Your task to perform on an android device: What's the news in theFalkland Islands? Image 0: 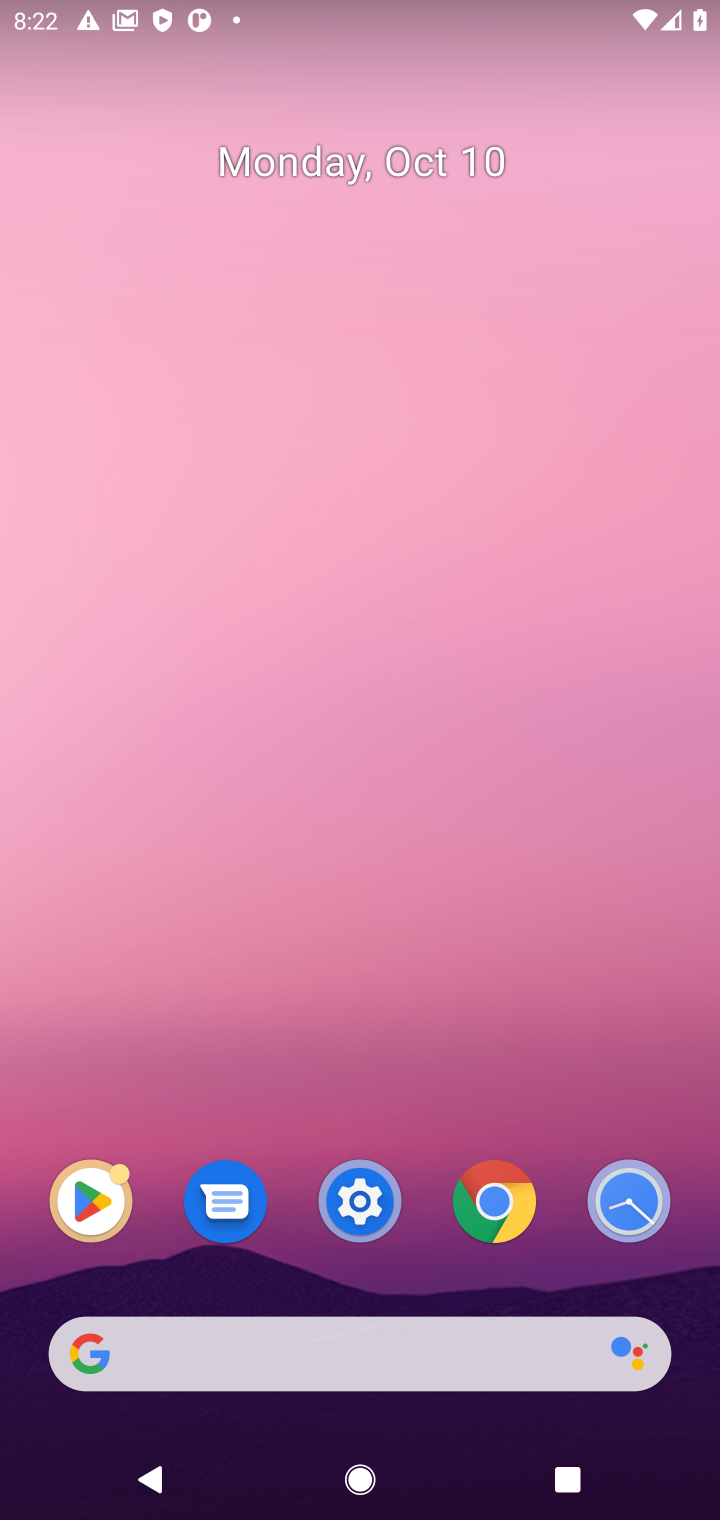
Step 0: click (474, 1193)
Your task to perform on an android device: What's the news in theFalkland Islands? Image 1: 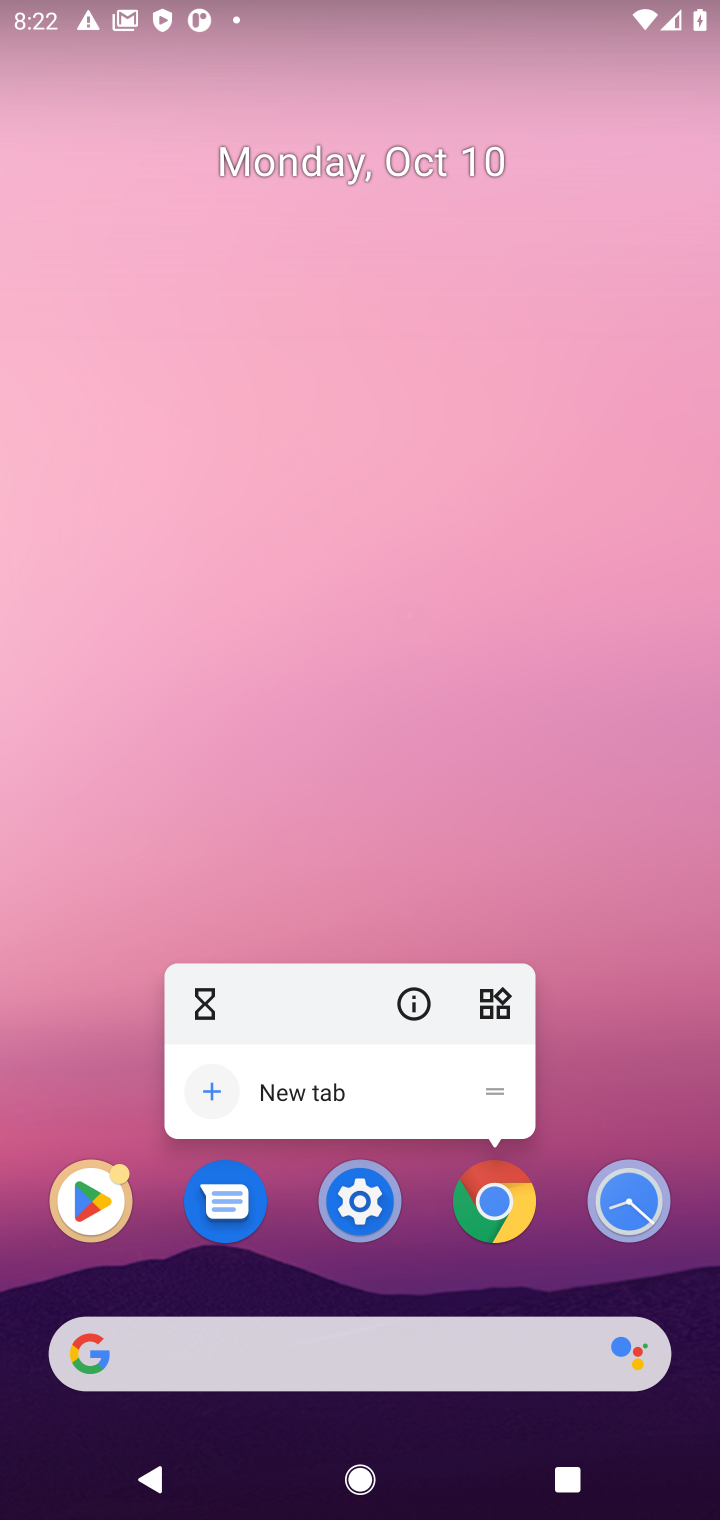
Step 1: click (490, 1201)
Your task to perform on an android device: What's the news in theFalkland Islands? Image 2: 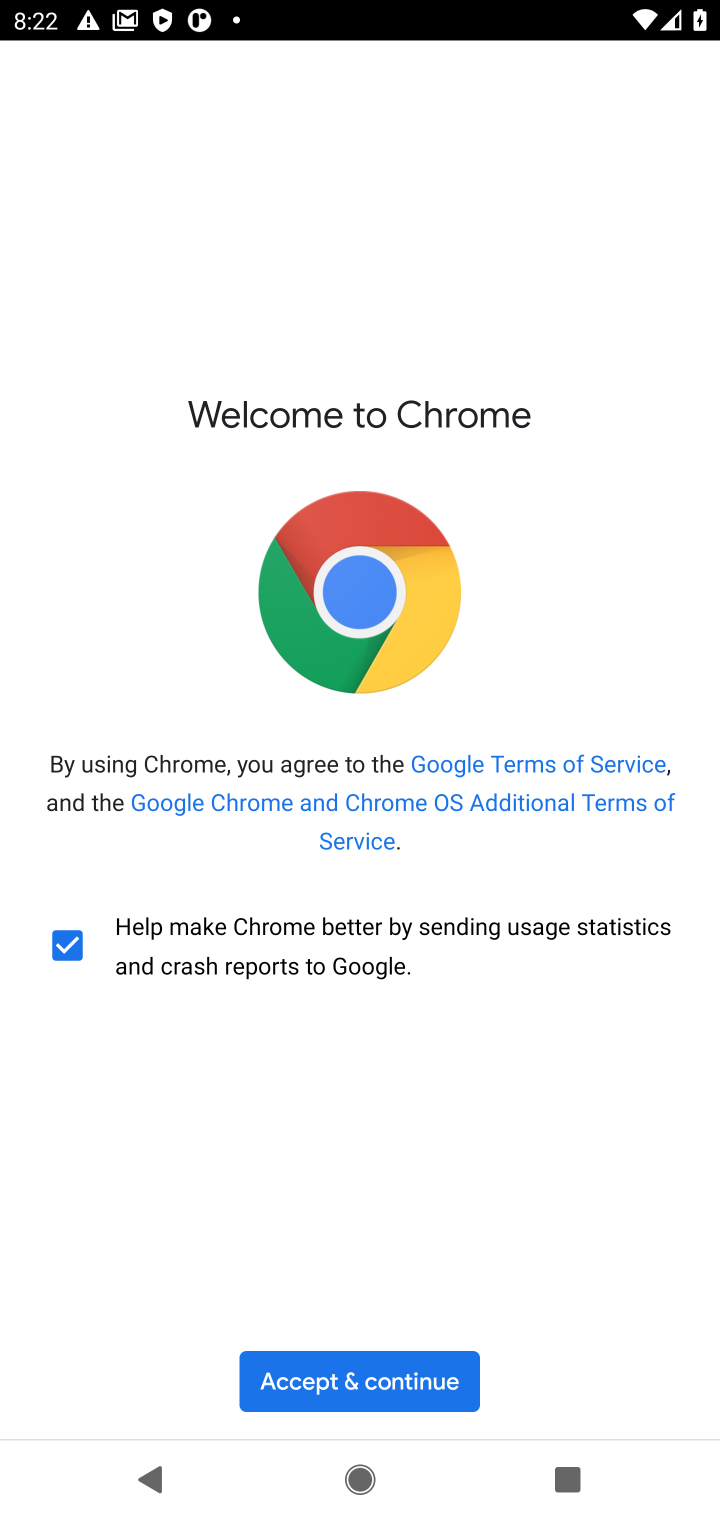
Step 2: click (368, 1375)
Your task to perform on an android device: What's the news in theFalkland Islands? Image 3: 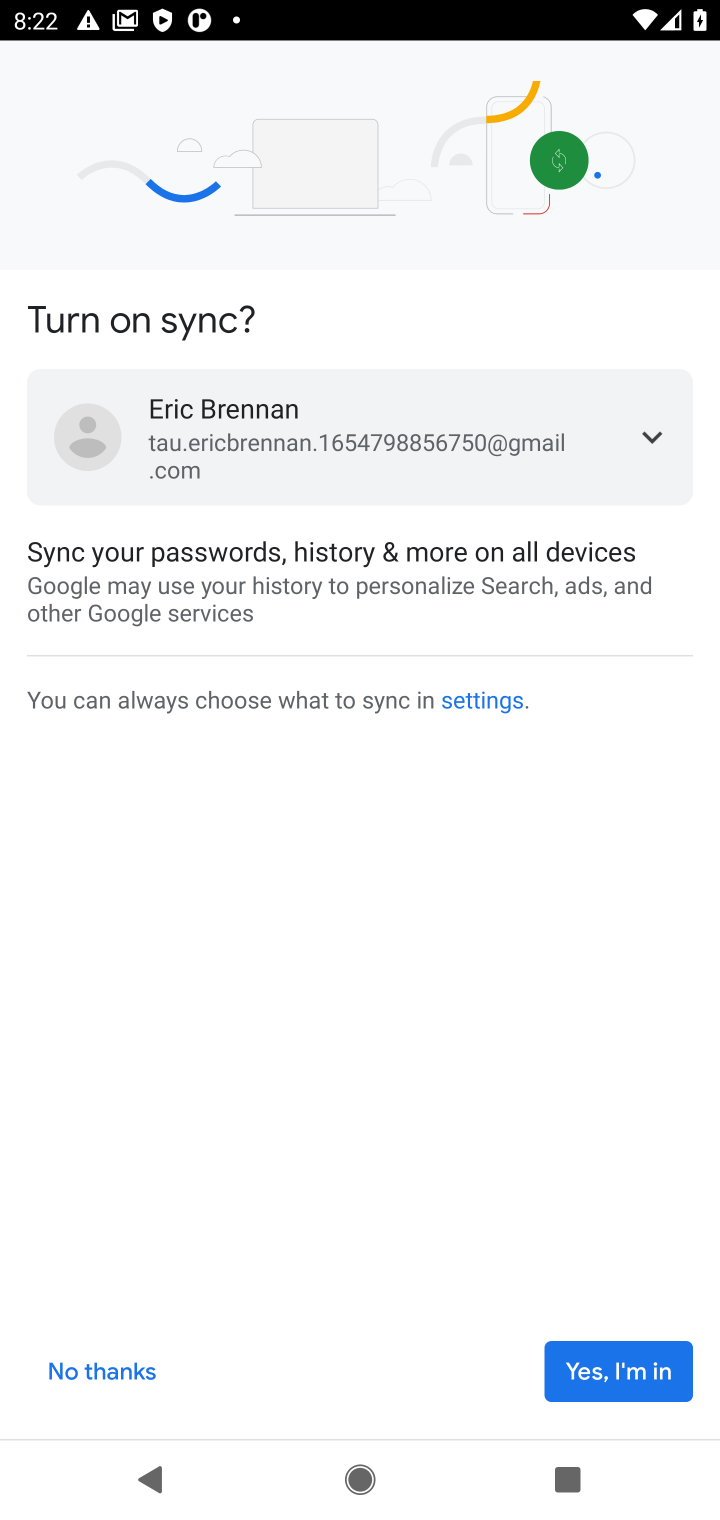
Step 3: click (550, 1349)
Your task to perform on an android device: What's the news in theFalkland Islands? Image 4: 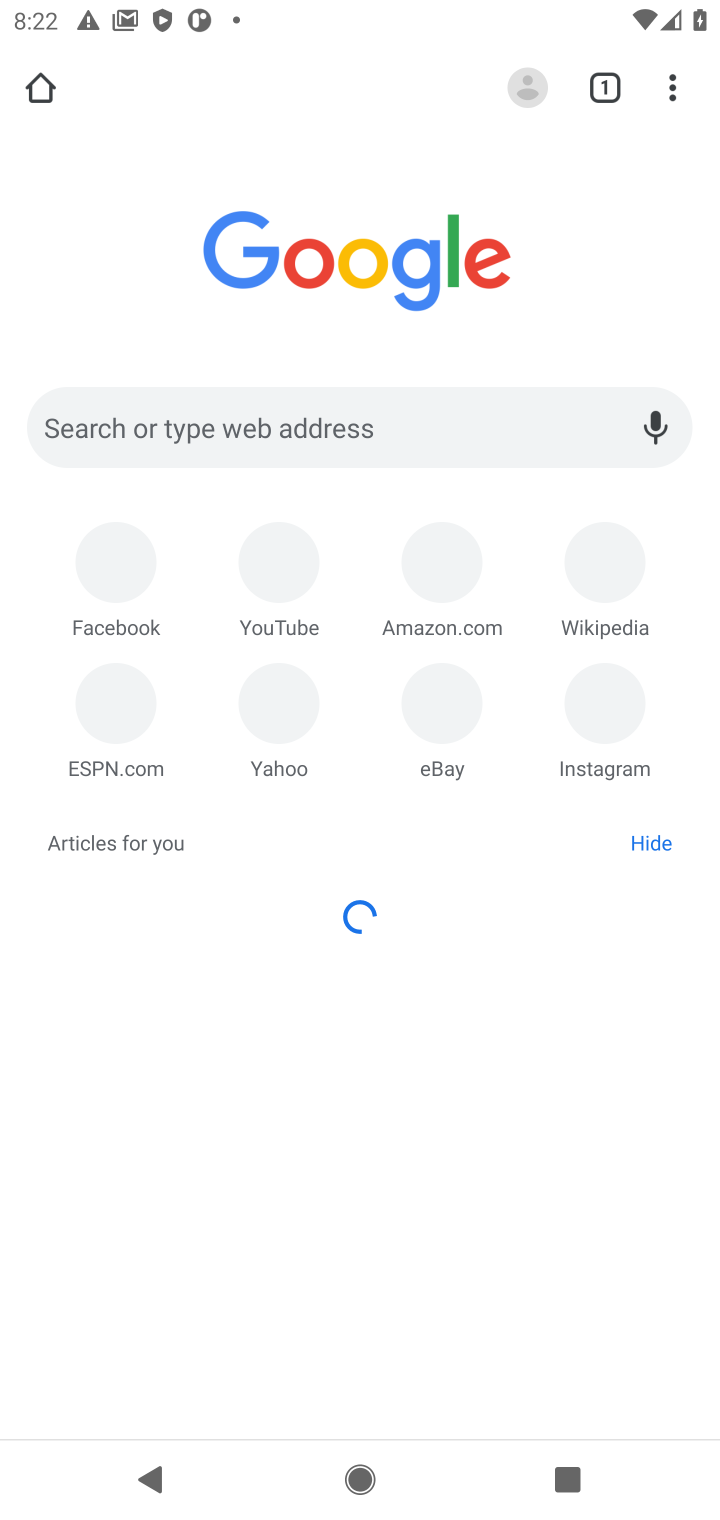
Step 4: click (197, 433)
Your task to perform on an android device: What's the news in theFalkland Islands? Image 5: 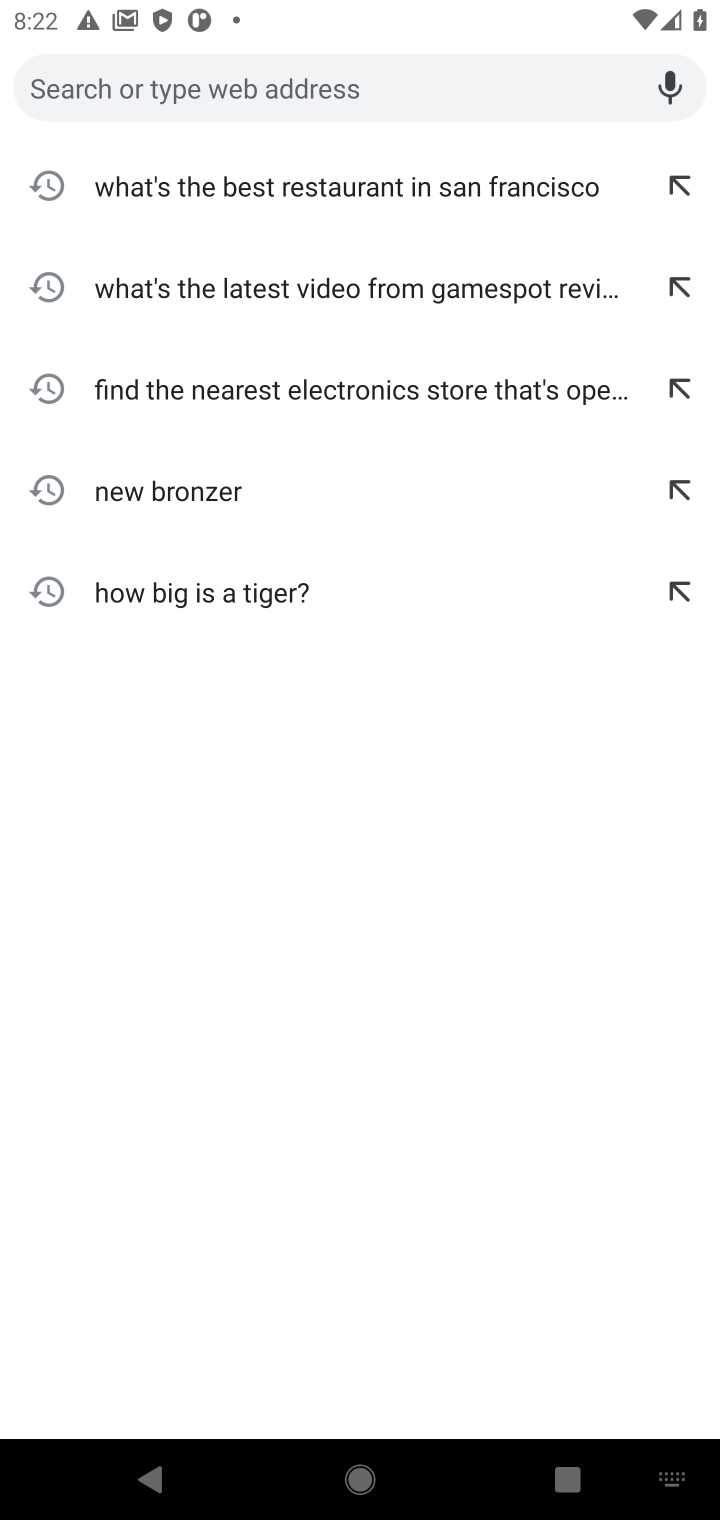
Step 5: type "What's the news in theFalkland Islands?"
Your task to perform on an android device: What's the news in theFalkland Islands? Image 6: 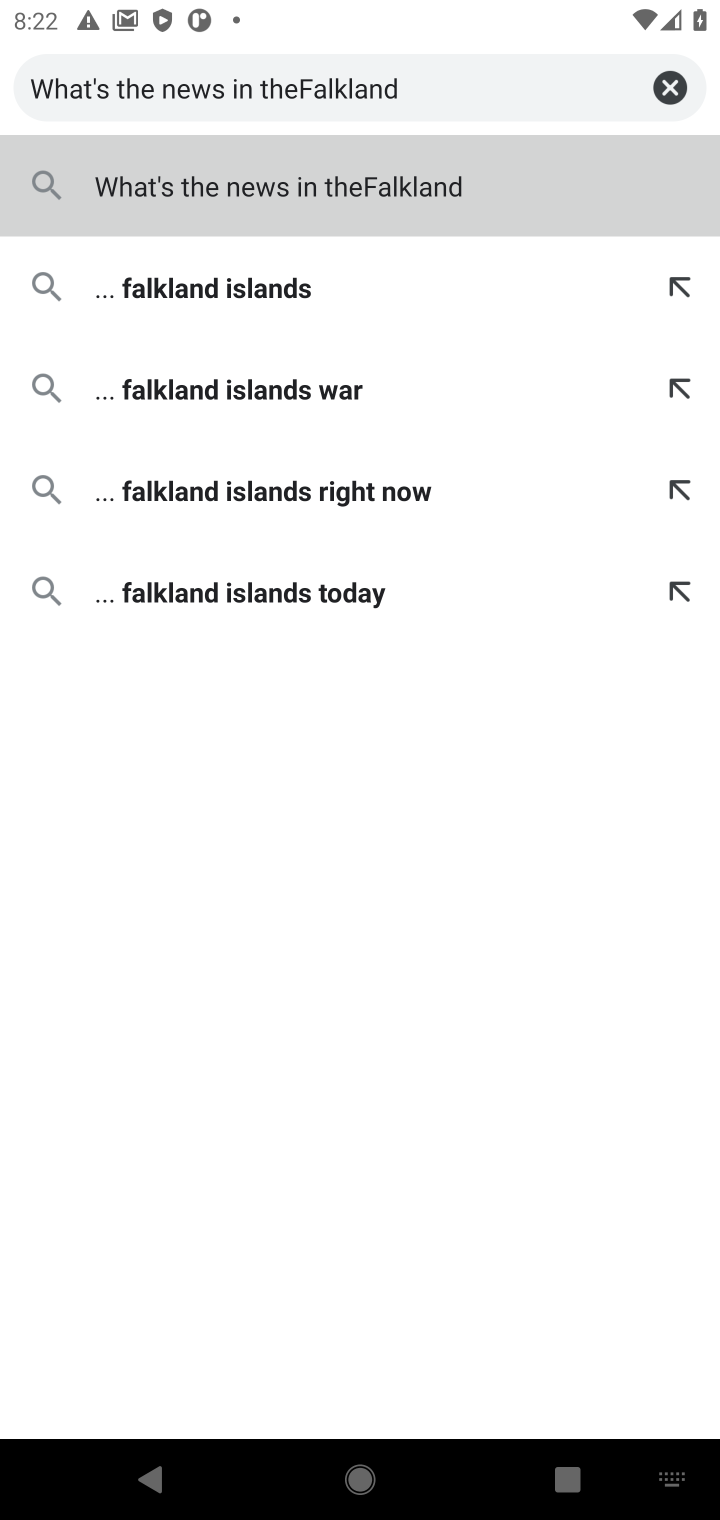
Step 6: type ""
Your task to perform on an android device: What's the news in theFalkland Islands? Image 7: 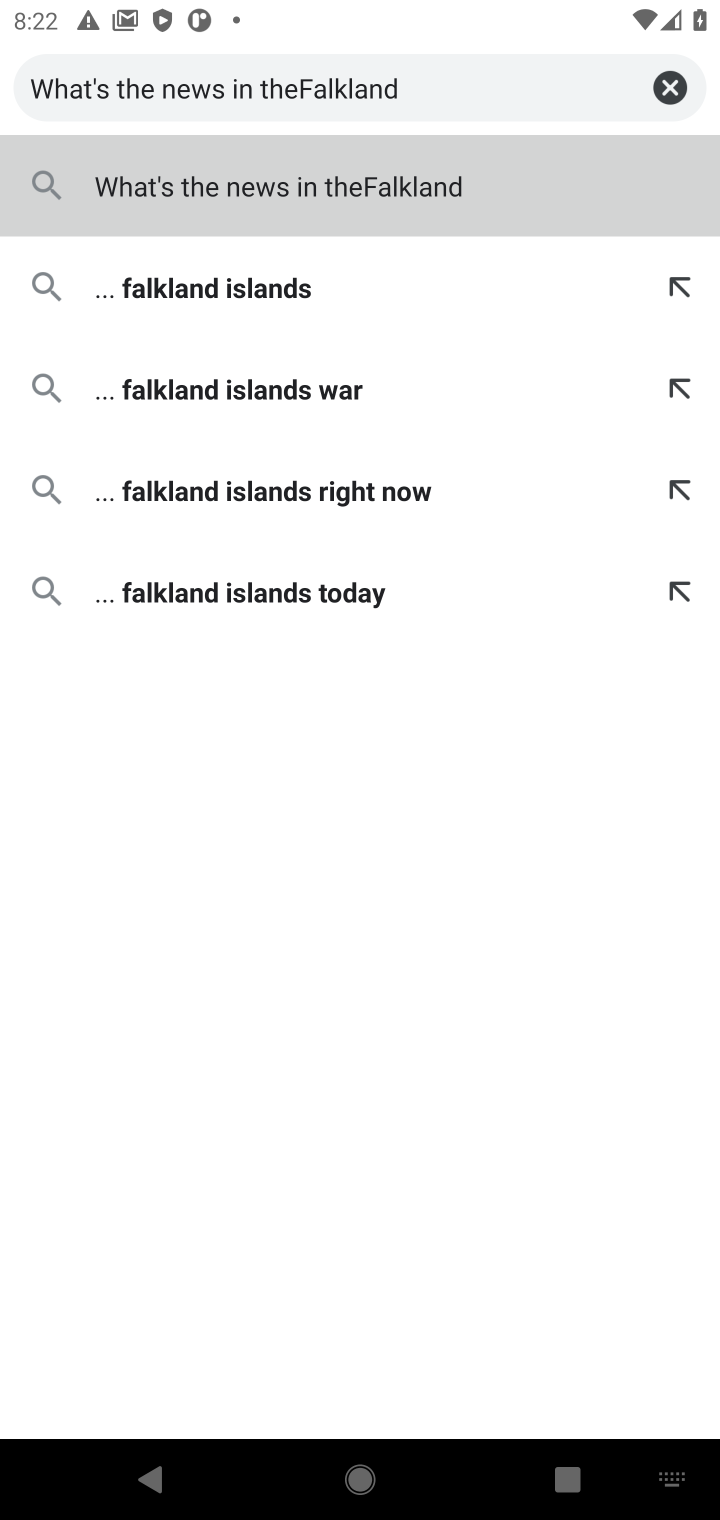
Step 7: click (369, 185)
Your task to perform on an android device: What's the news in theFalkland Islands? Image 8: 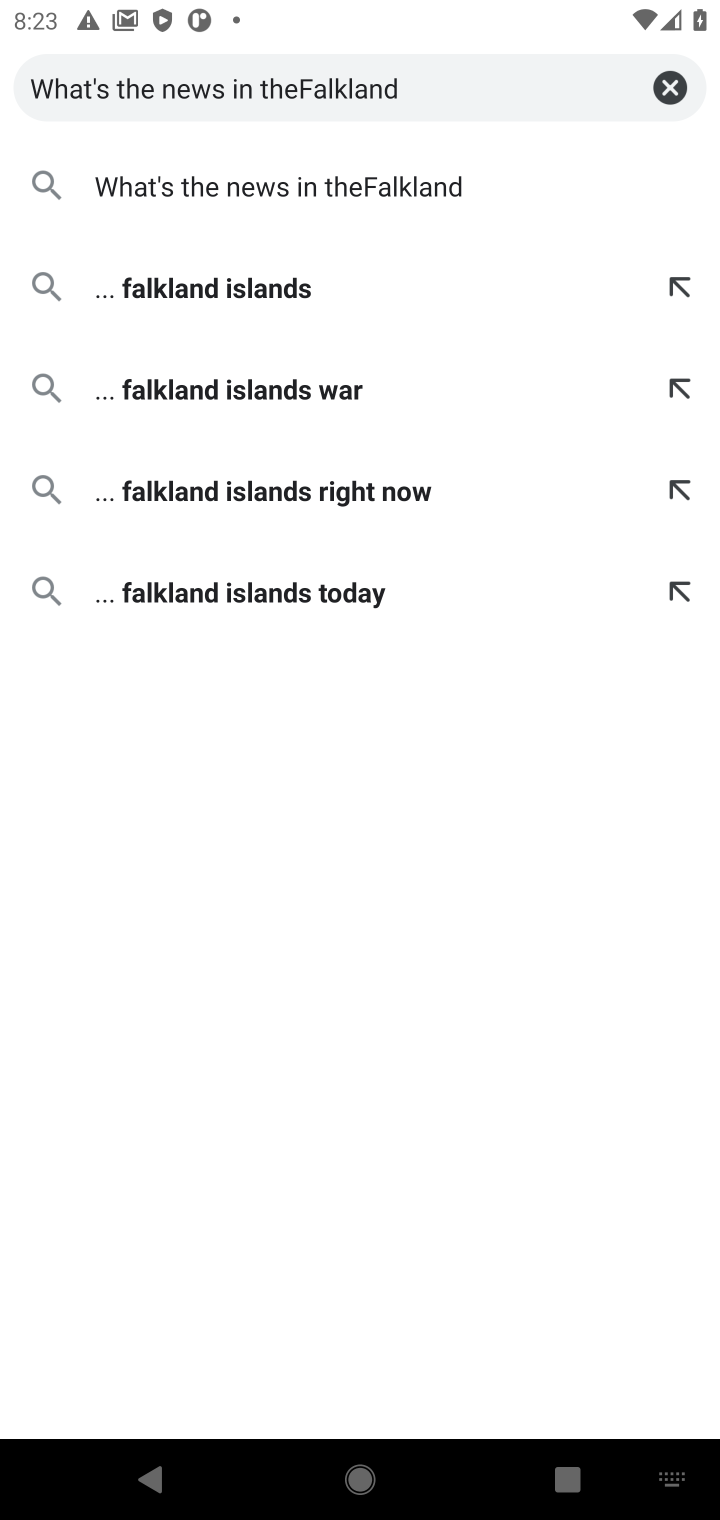
Step 8: click (369, 185)
Your task to perform on an android device: What's the news in theFalkland Islands? Image 9: 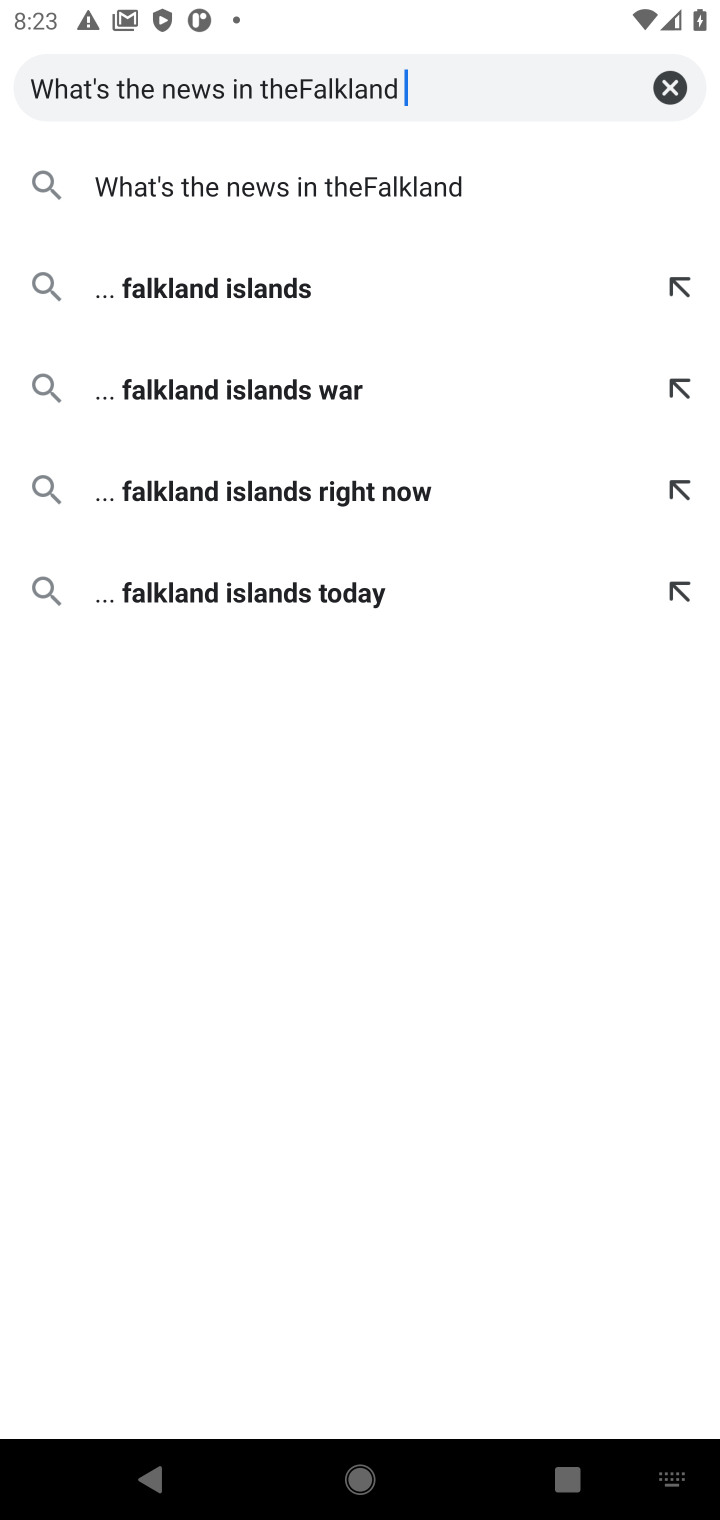
Step 9: press enter
Your task to perform on an android device: What's the news in theFalkland Islands? Image 10: 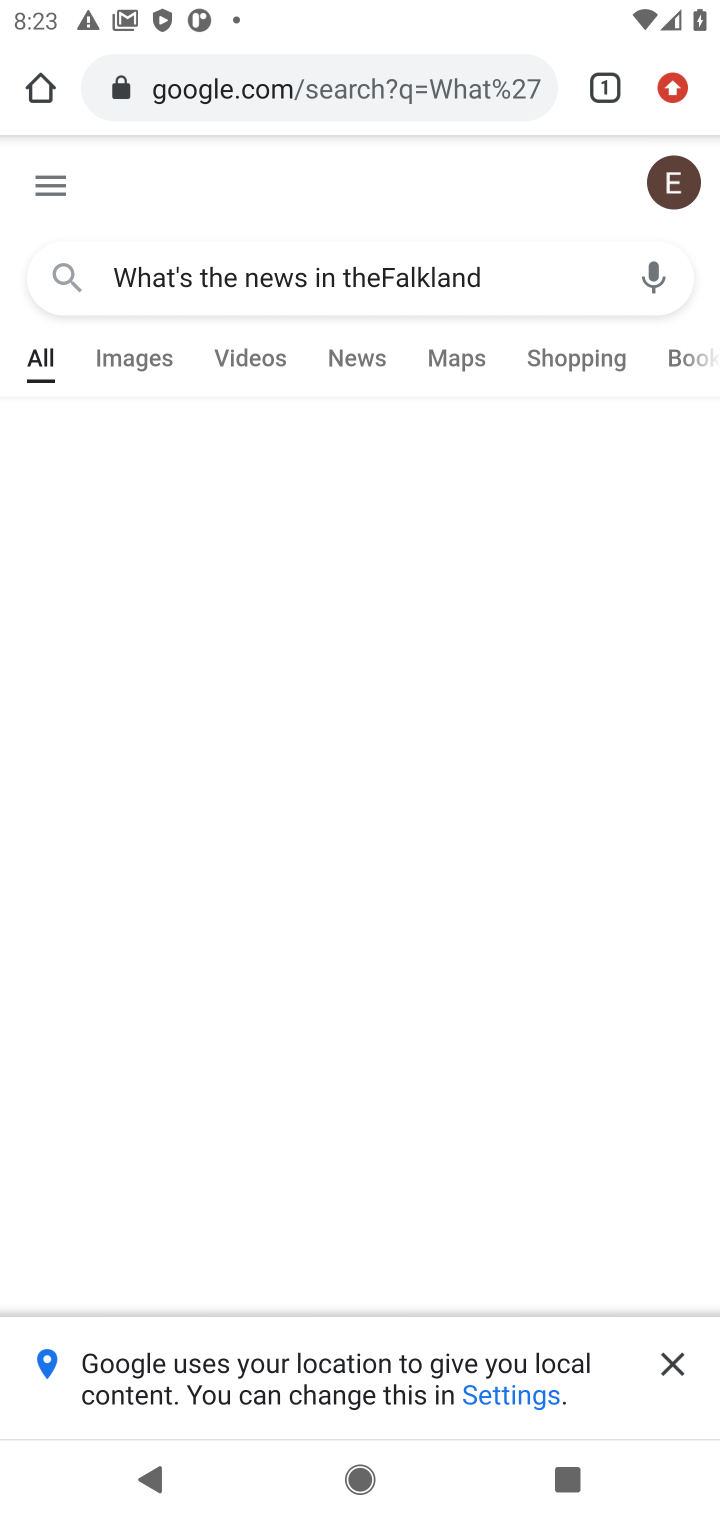
Step 10: click (669, 1370)
Your task to perform on an android device: What's the news in theFalkland Islands? Image 11: 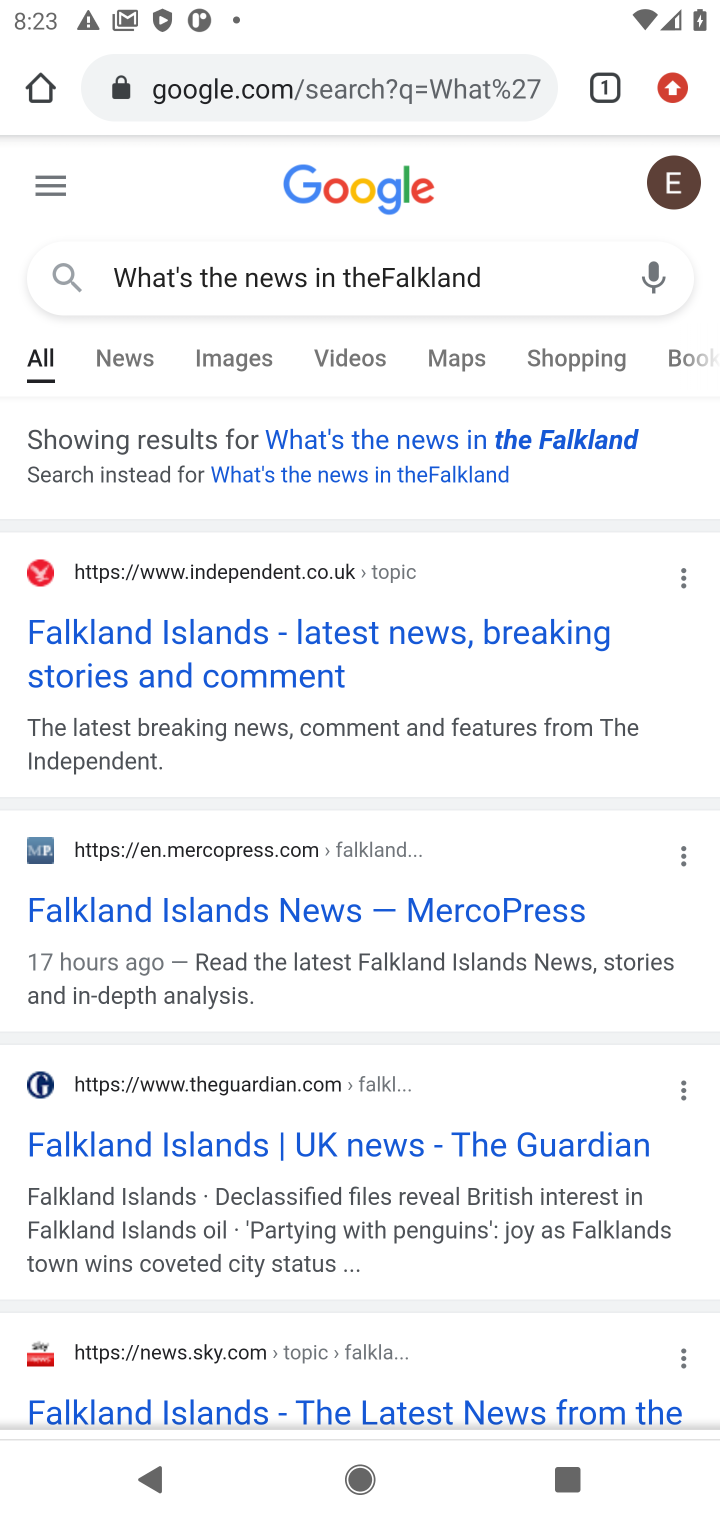
Step 11: drag from (336, 1180) to (460, 289)
Your task to perform on an android device: What's the news in theFalkland Islands? Image 12: 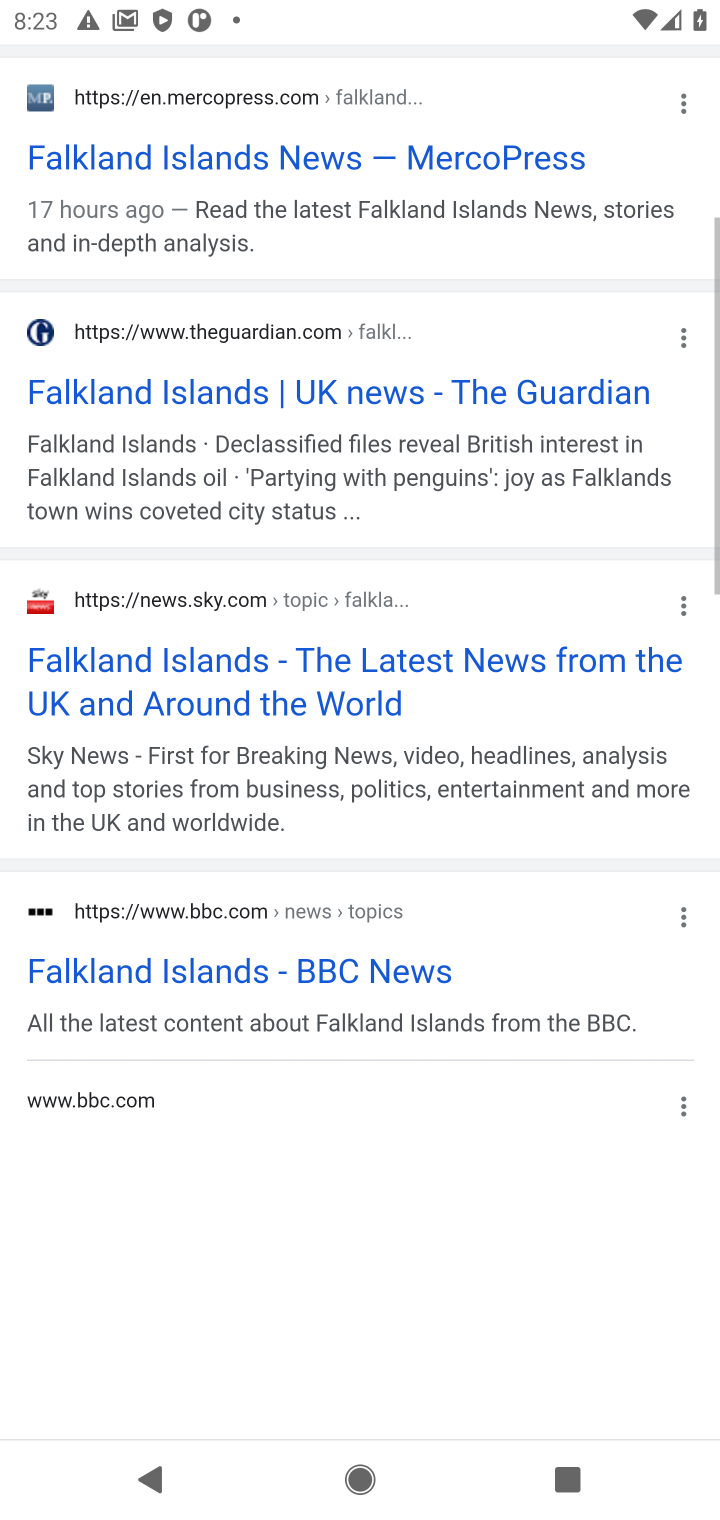
Step 12: drag from (228, 831) to (306, 476)
Your task to perform on an android device: What's the news in theFalkland Islands? Image 13: 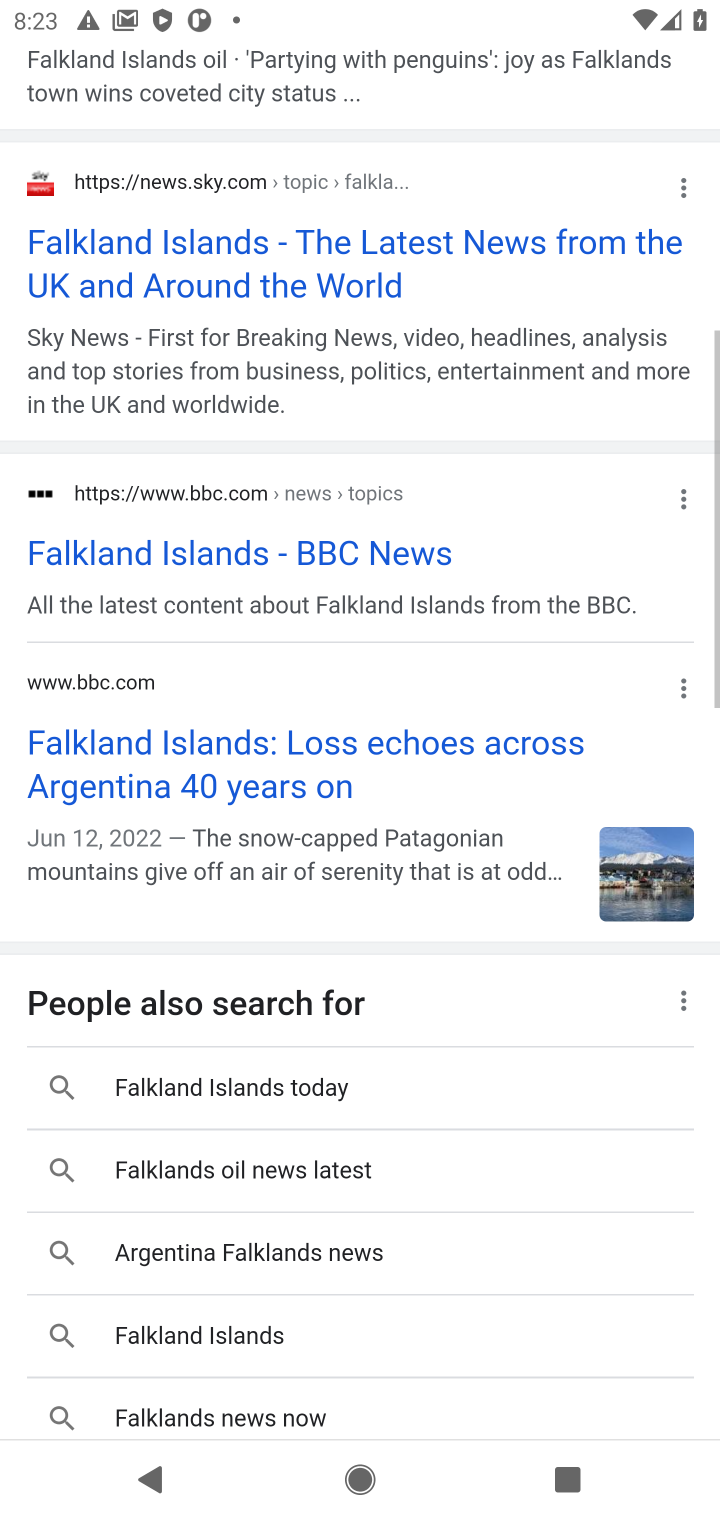
Step 13: drag from (358, 744) to (334, 1272)
Your task to perform on an android device: What's the news in theFalkland Islands? Image 14: 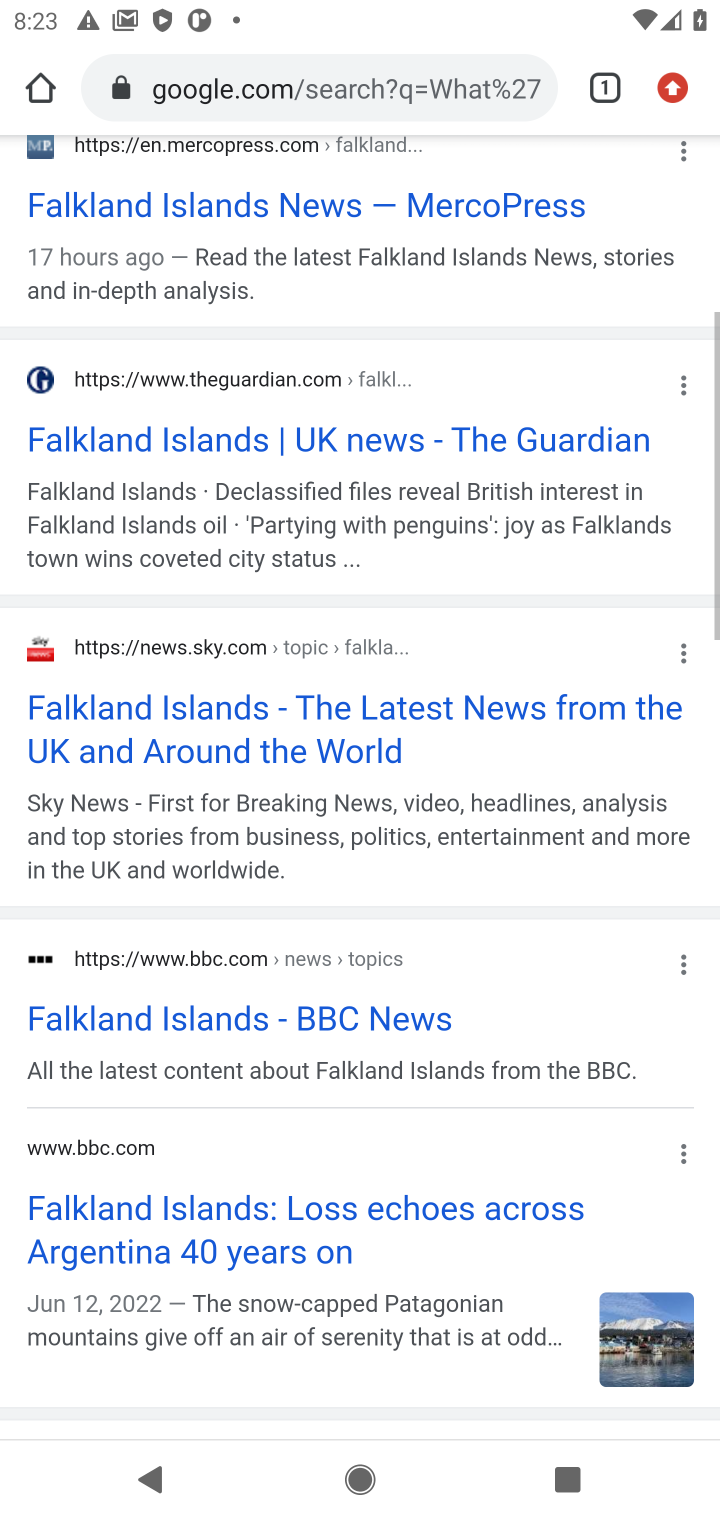
Step 14: drag from (373, 1301) to (373, 1373)
Your task to perform on an android device: What's the news in theFalkland Islands? Image 15: 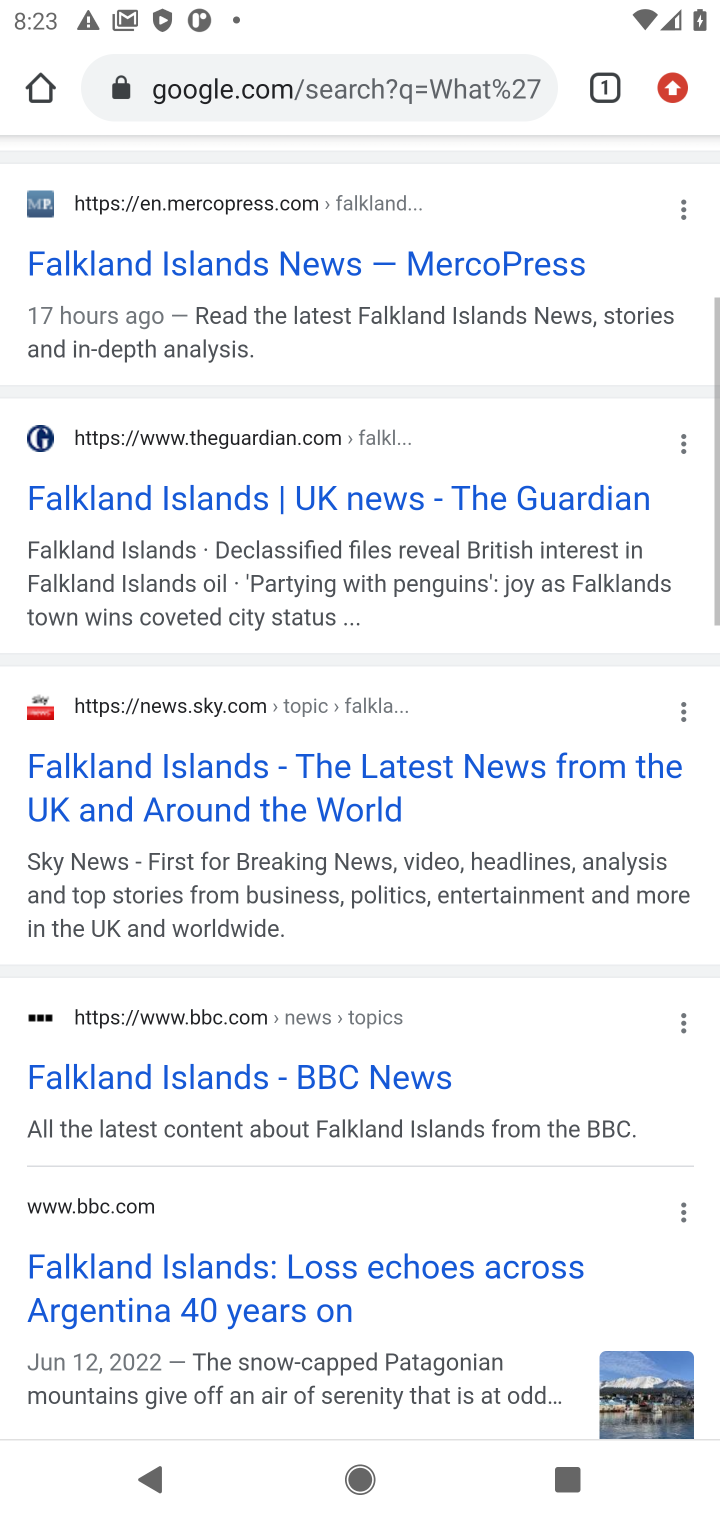
Step 15: click (401, 1296)
Your task to perform on an android device: What's the news in theFalkland Islands? Image 16: 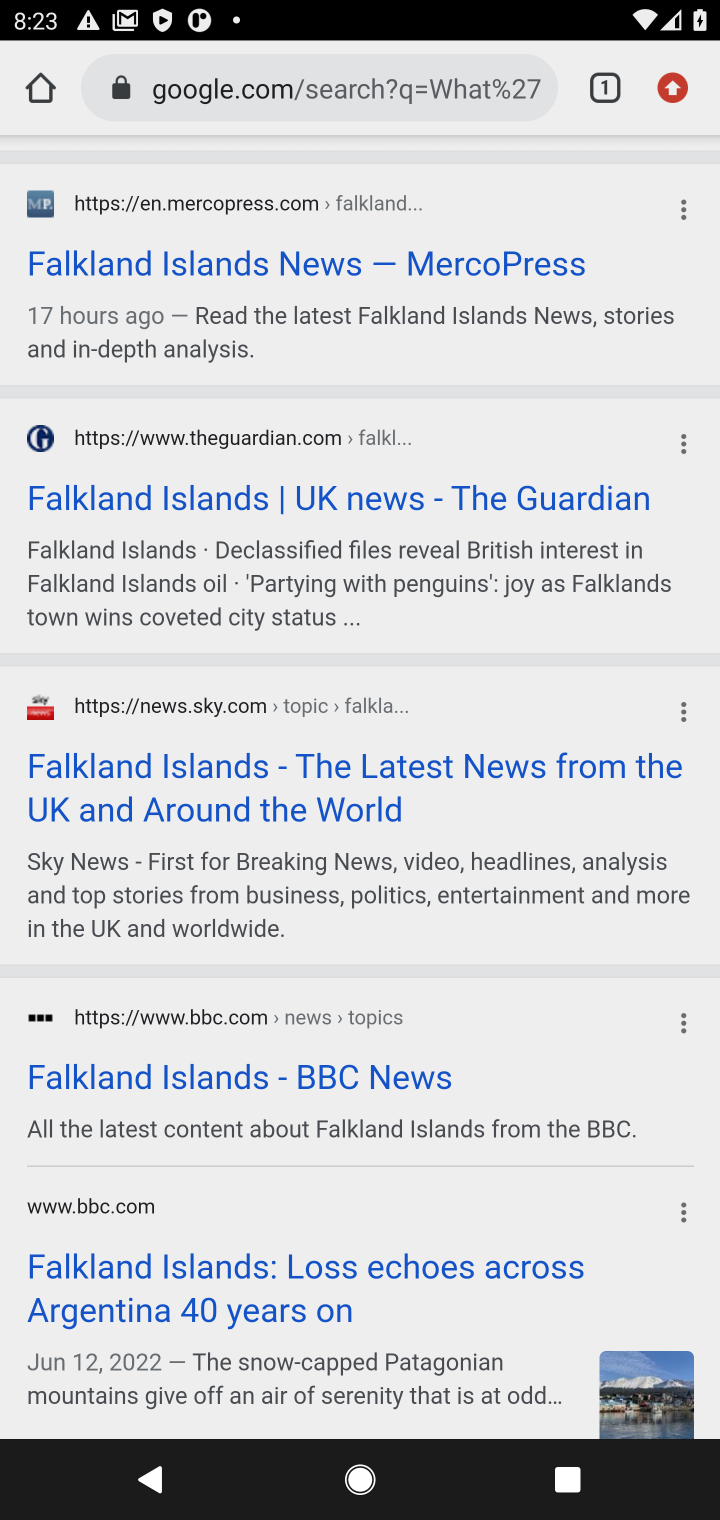
Step 16: click (204, 488)
Your task to perform on an android device: What's the news in theFalkland Islands? Image 17: 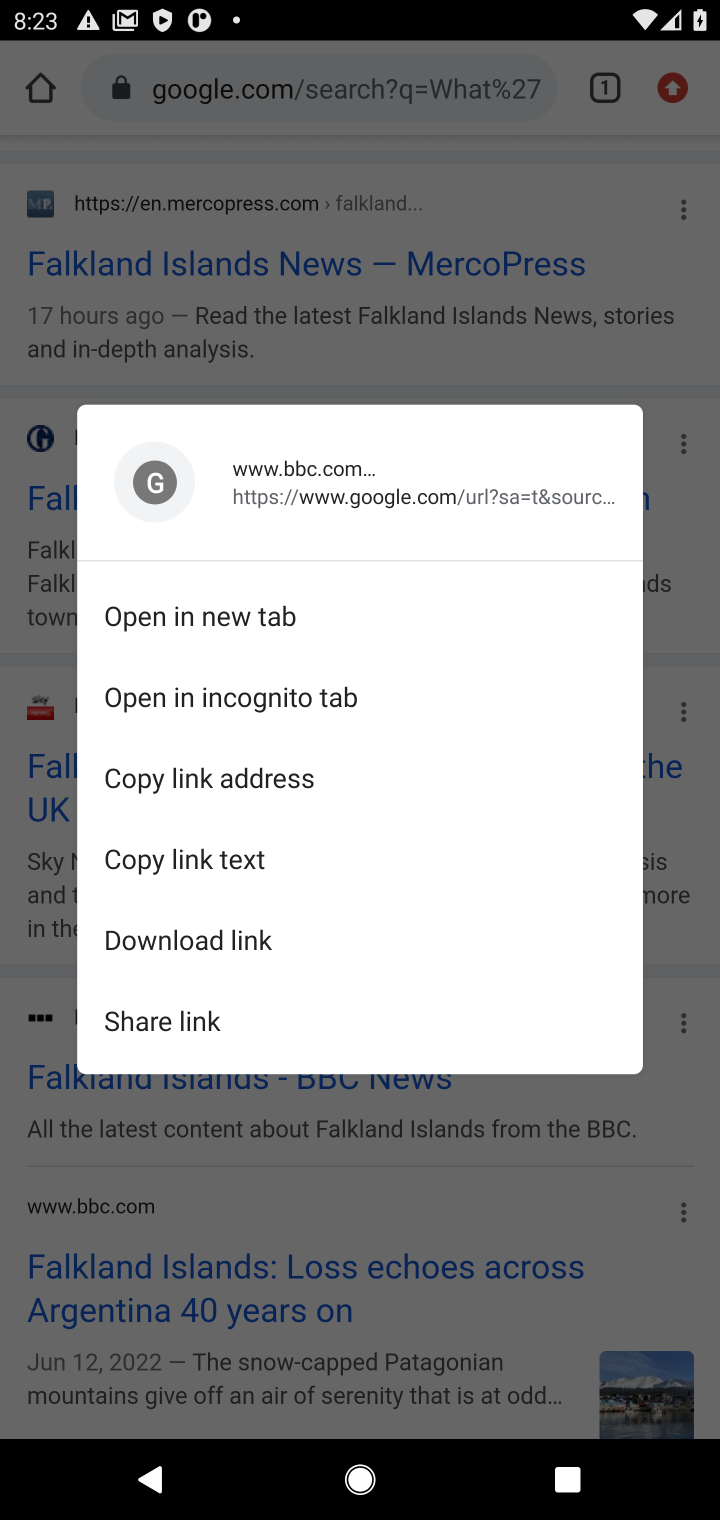
Step 17: click (272, 339)
Your task to perform on an android device: What's the news in theFalkland Islands? Image 18: 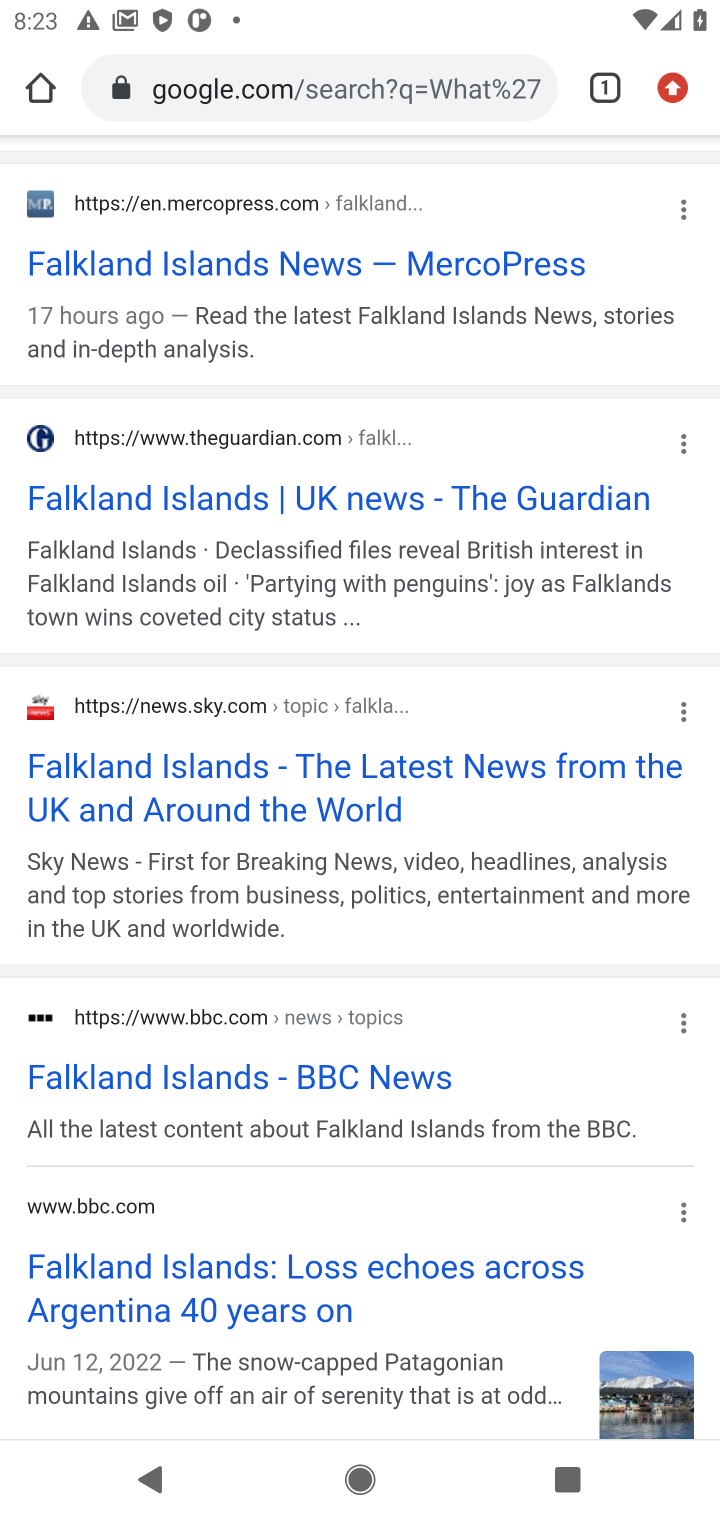
Step 18: click (214, 504)
Your task to perform on an android device: What's the news in theFalkland Islands? Image 19: 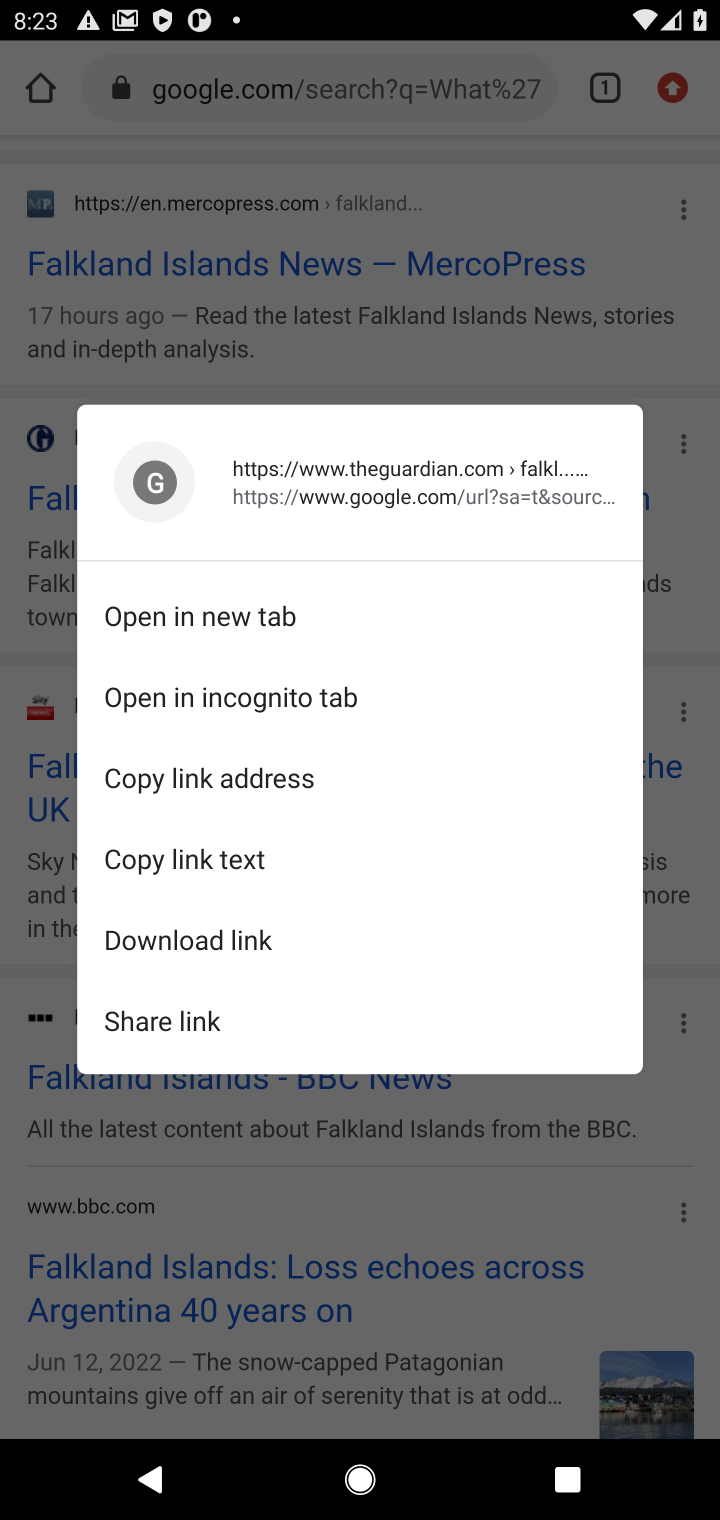
Step 19: click (339, 279)
Your task to perform on an android device: What's the news in theFalkland Islands? Image 20: 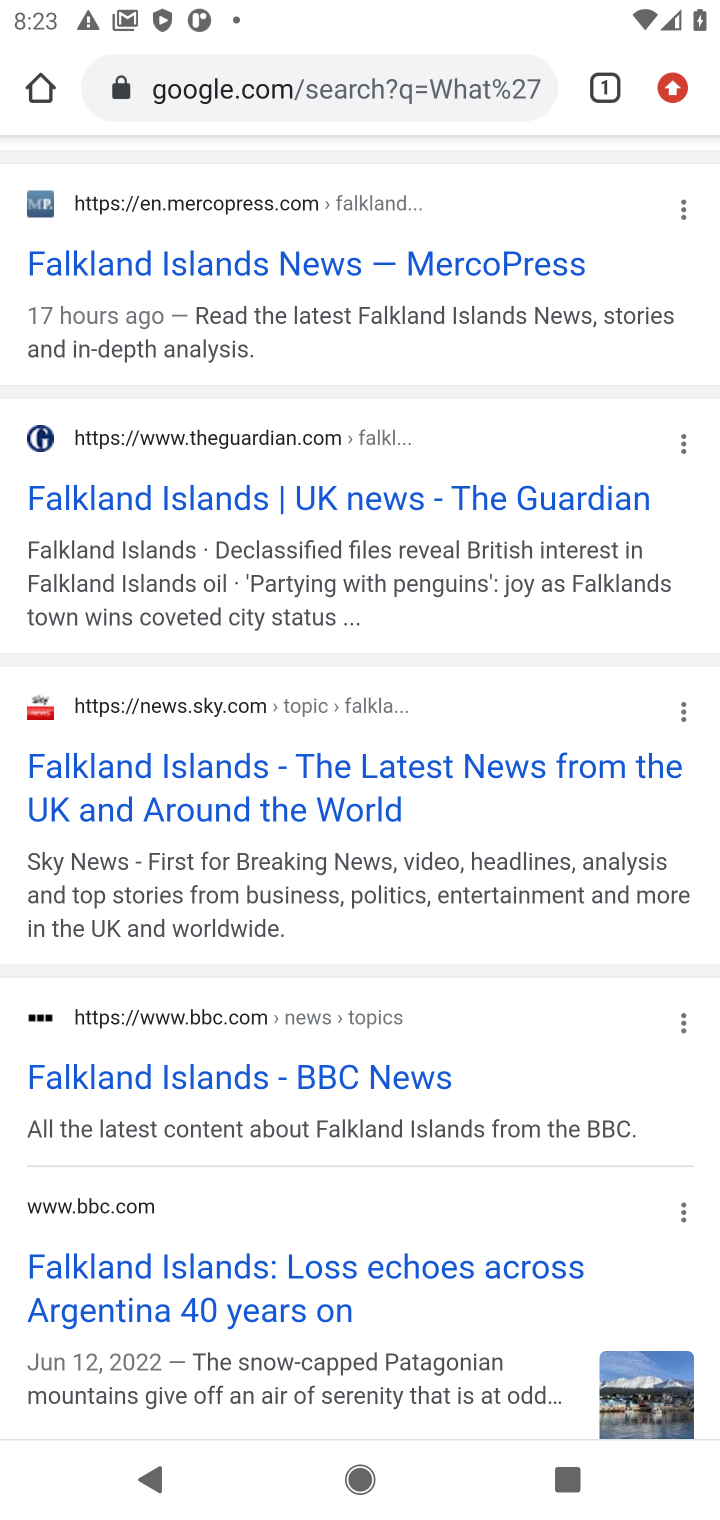
Step 20: click (286, 275)
Your task to perform on an android device: What's the news in theFalkland Islands? Image 21: 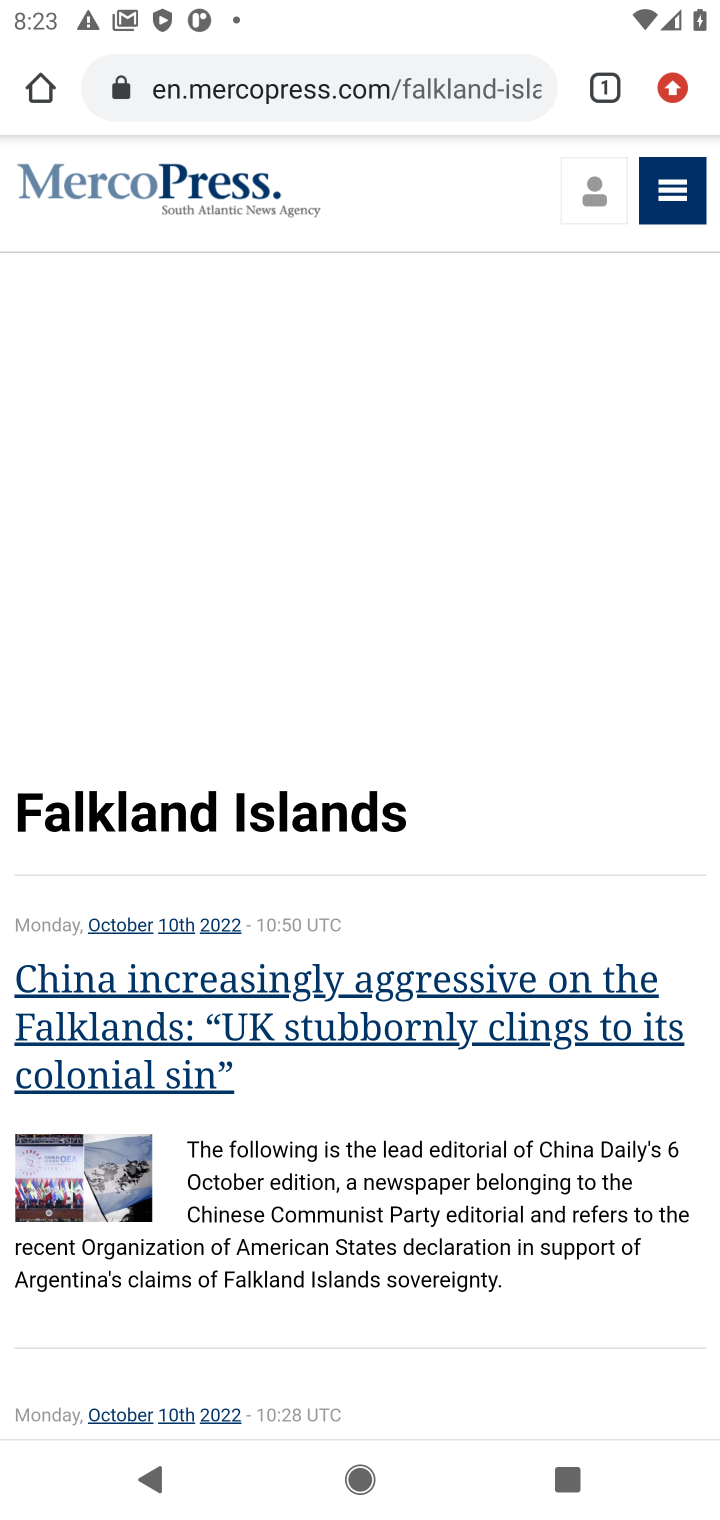
Step 21: drag from (253, 1159) to (346, 421)
Your task to perform on an android device: What's the news in theFalkland Islands? Image 22: 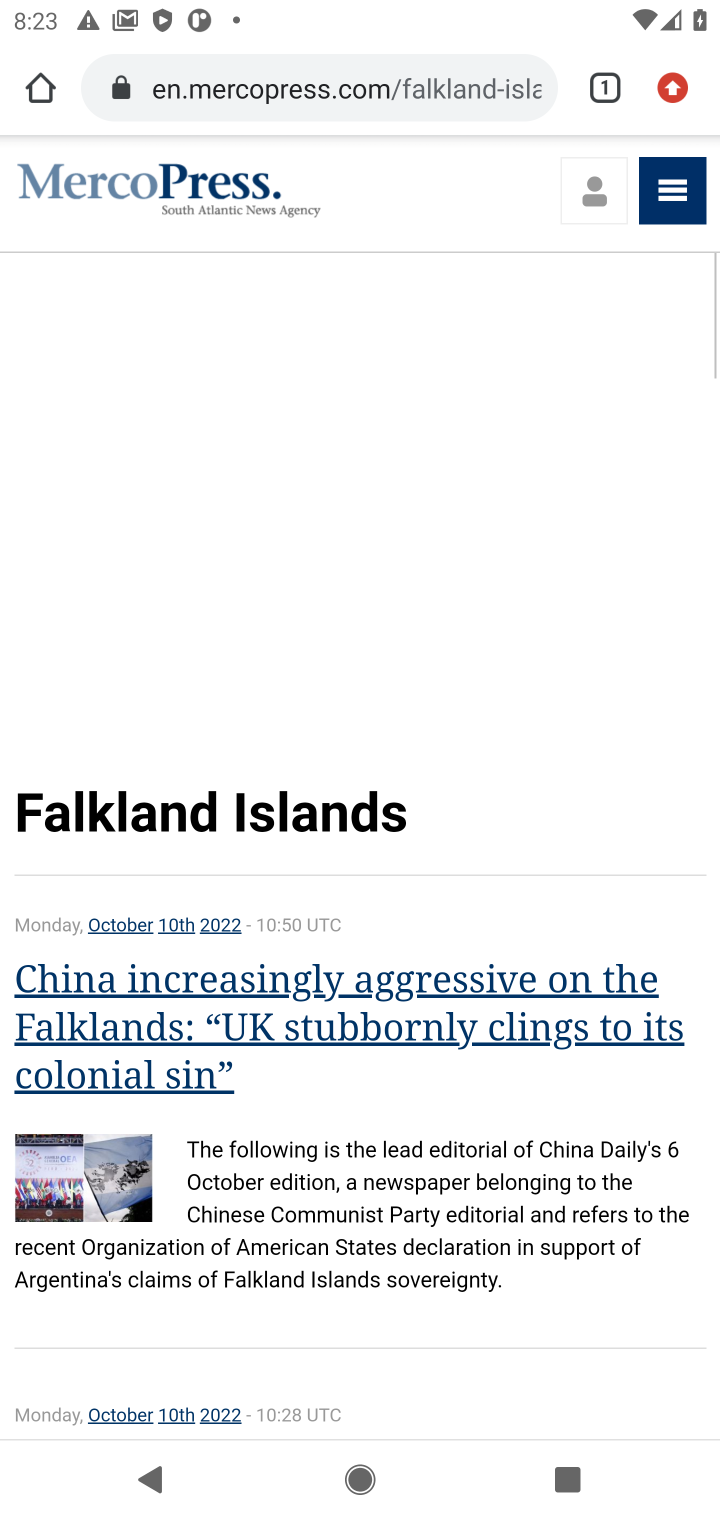
Step 22: drag from (222, 478) to (321, 372)
Your task to perform on an android device: What's the news in theFalkland Islands? Image 23: 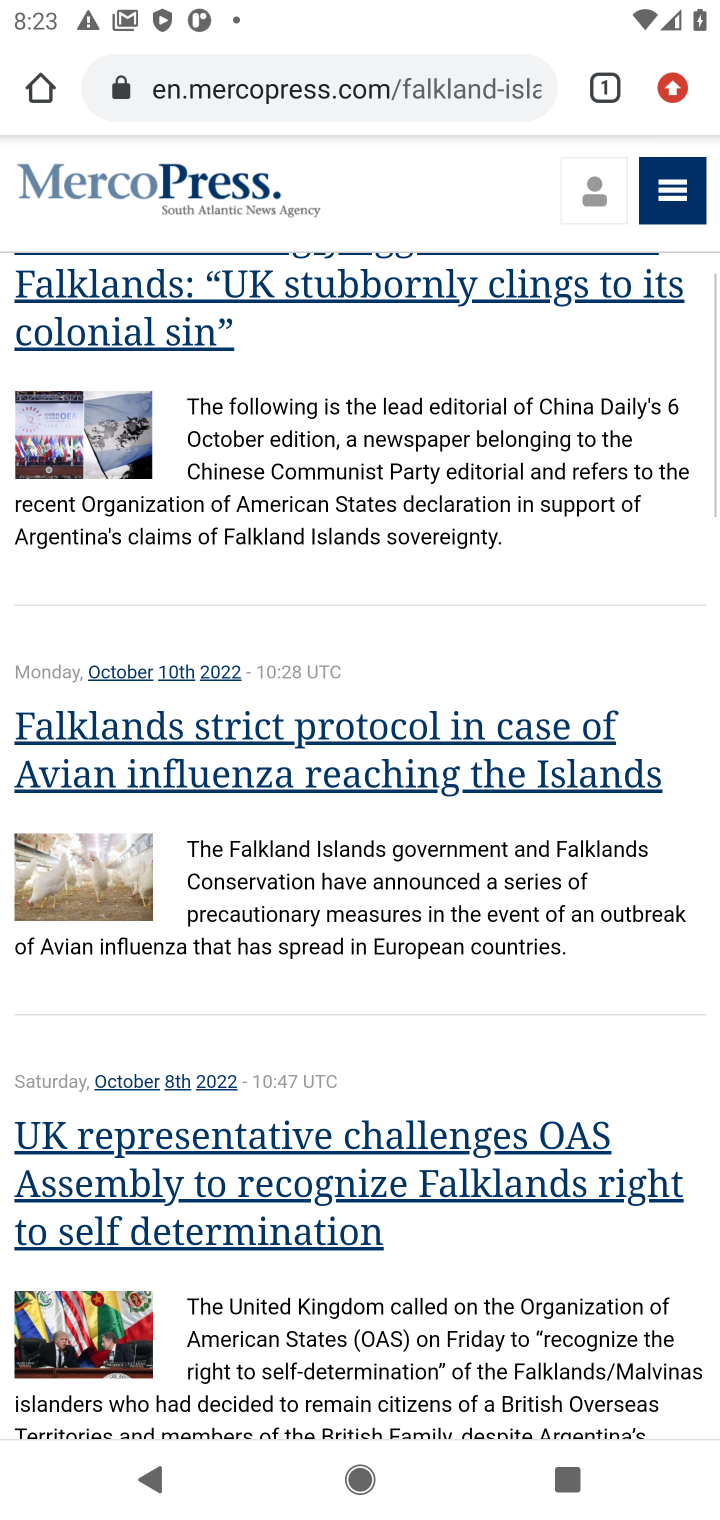
Step 23: click (369, 362)
Your task to perform on an android device: What's the news in theFalkland Islands? Image 24: 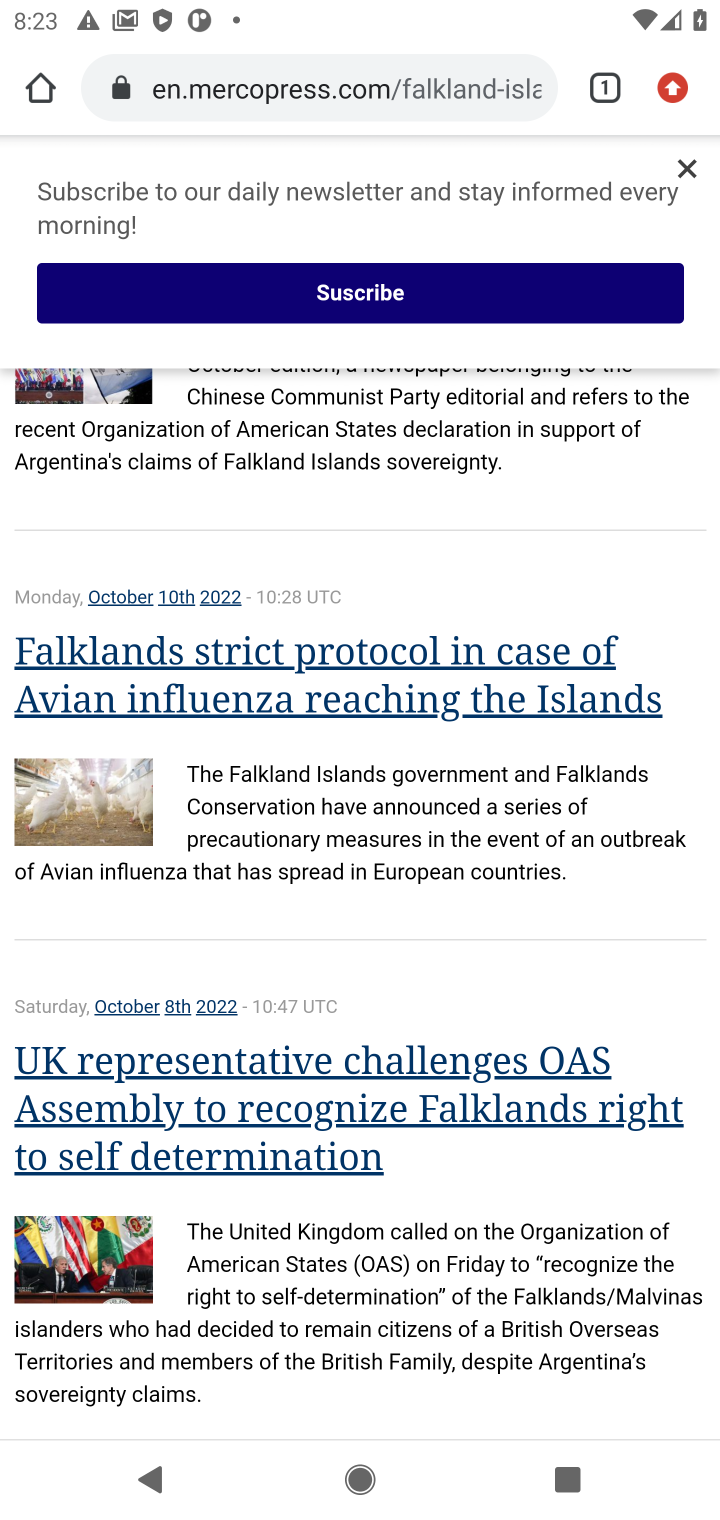
Step 24: click (389, 384)
Your task to perform on an android device: What's the news in theFalkland Islands? Image 25: 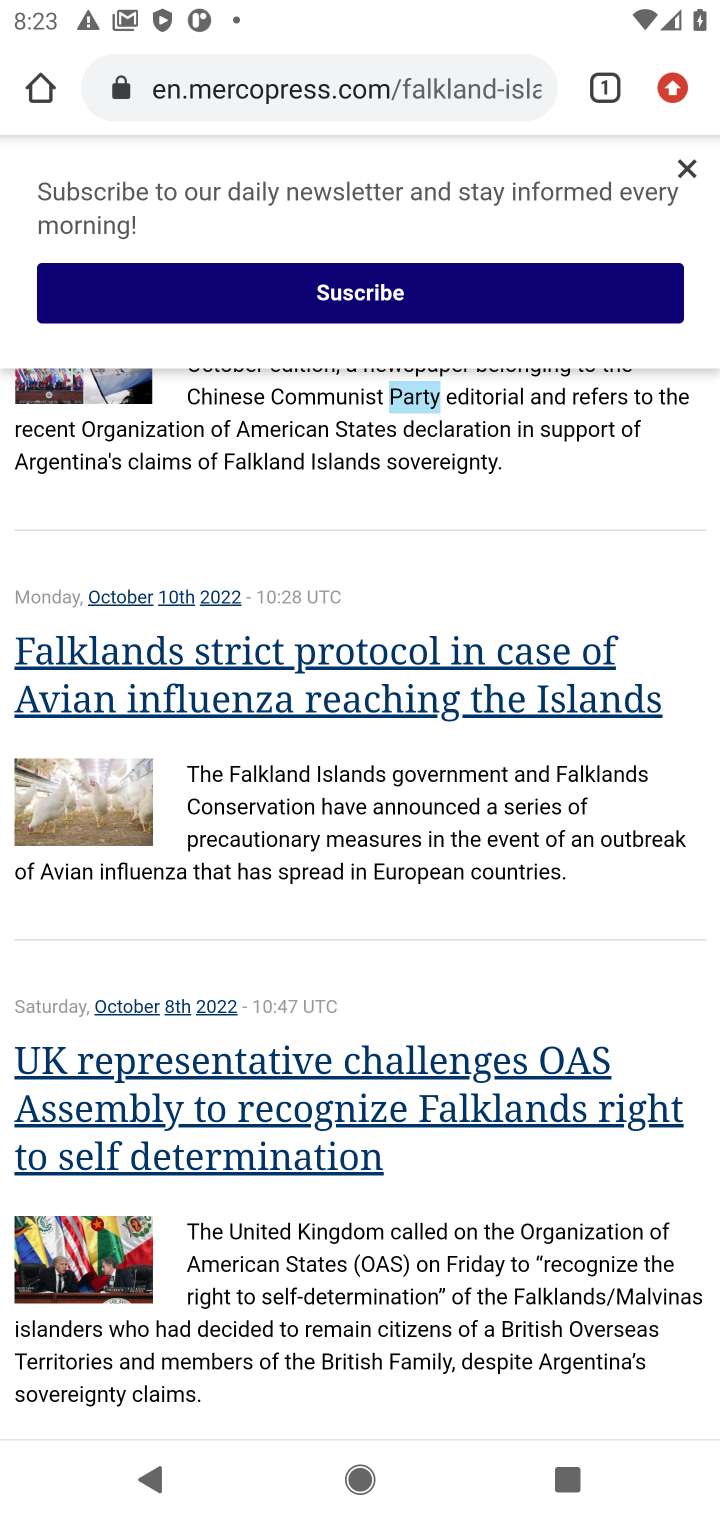
Step 25: drag from (341, 342) to (271, 468)
Your task to perform on an android device: What's the news in theFalkland Islands? Image 26: 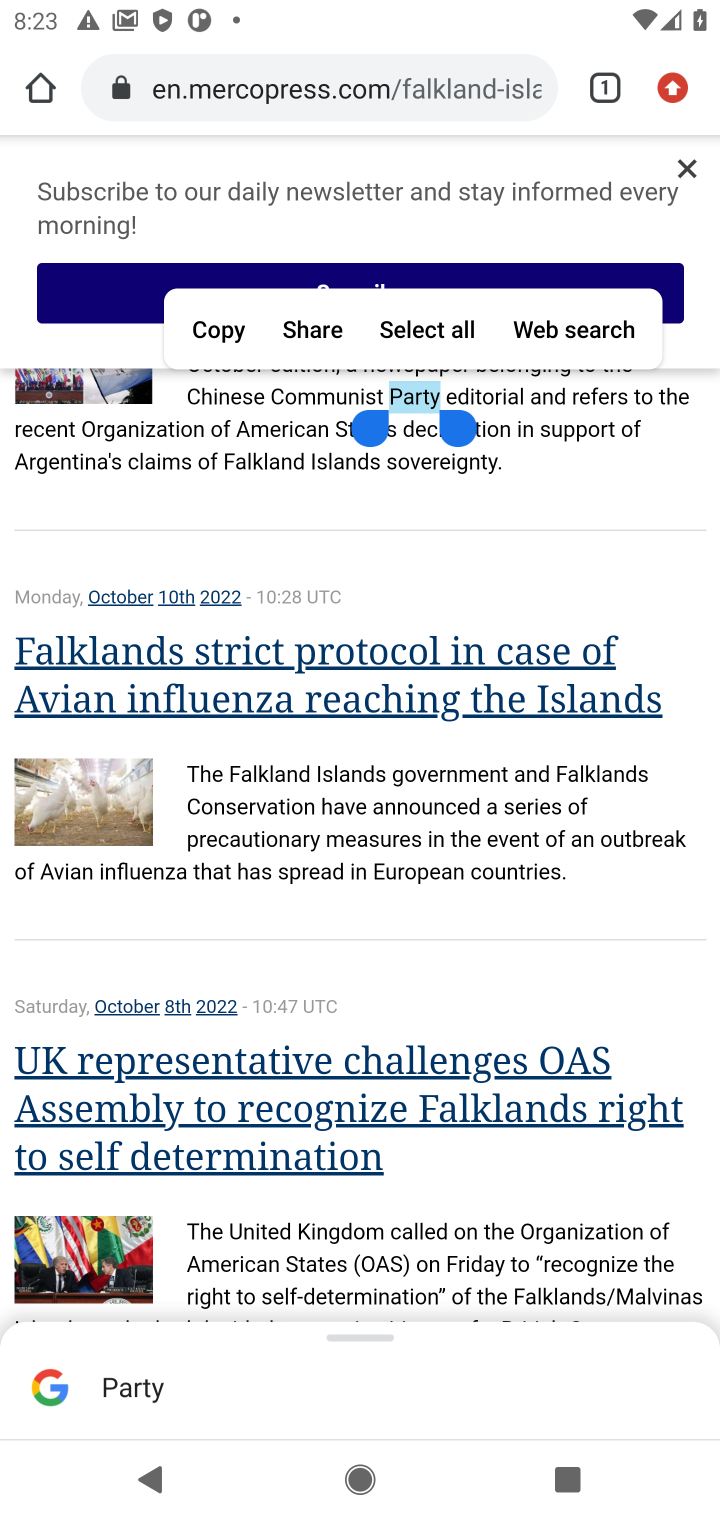
Step 26: press back button
Your task to perform on an android device: What's the news in theFalkland Islands? Image 27: 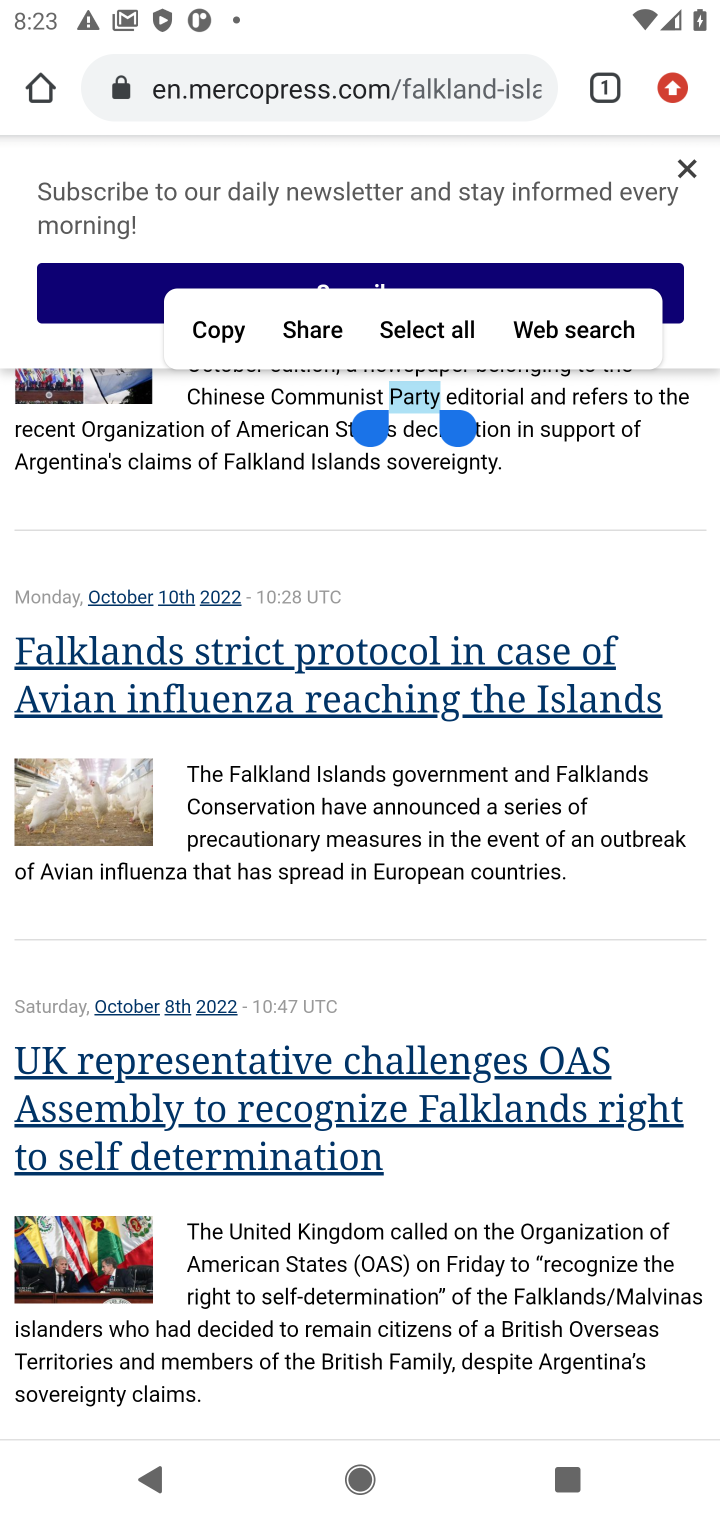
Step 27: click (384, 566)
Your task to perform on an android device: What's the news in theFalkland Islands? Image 28: 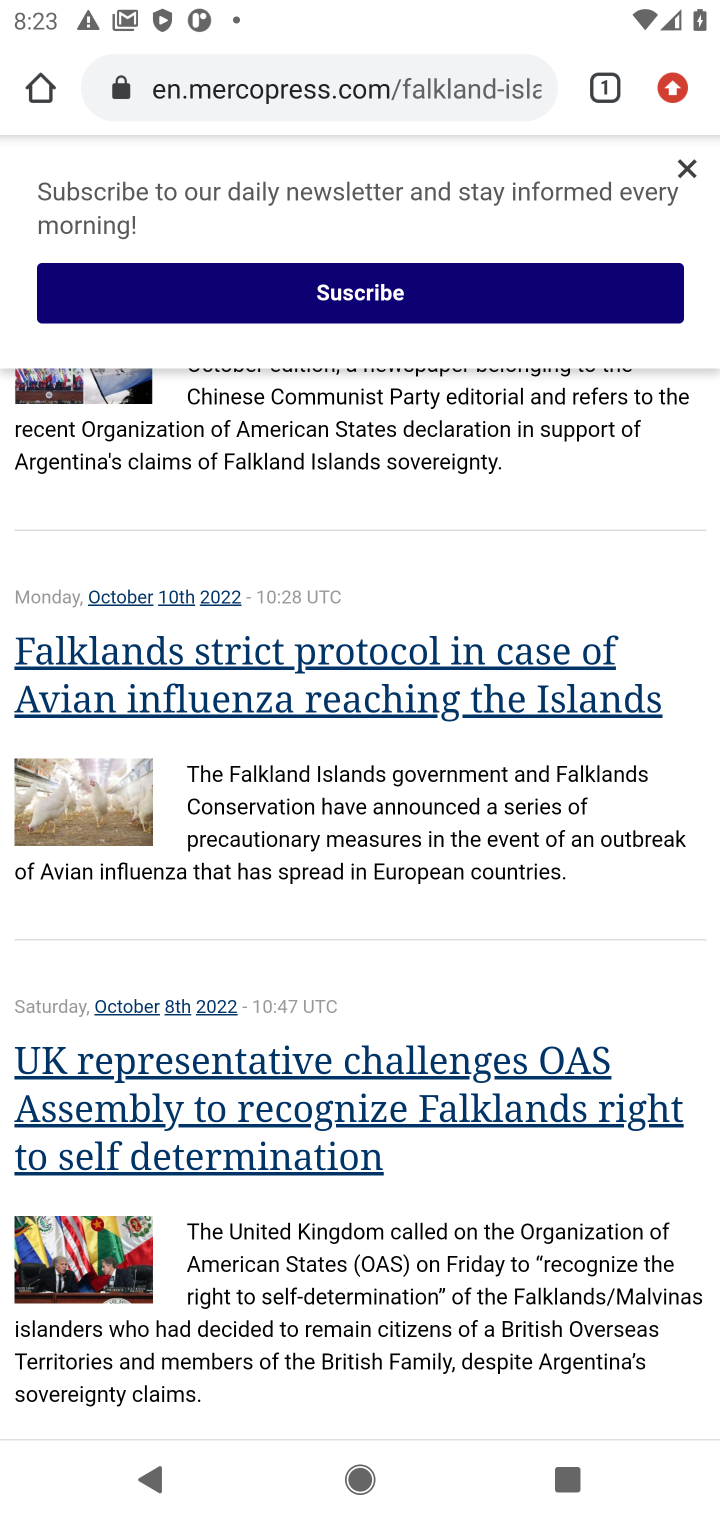
Step 28: press back button
Your task to perform on an android device: What's the news in theFalkland Islands? Image 29: 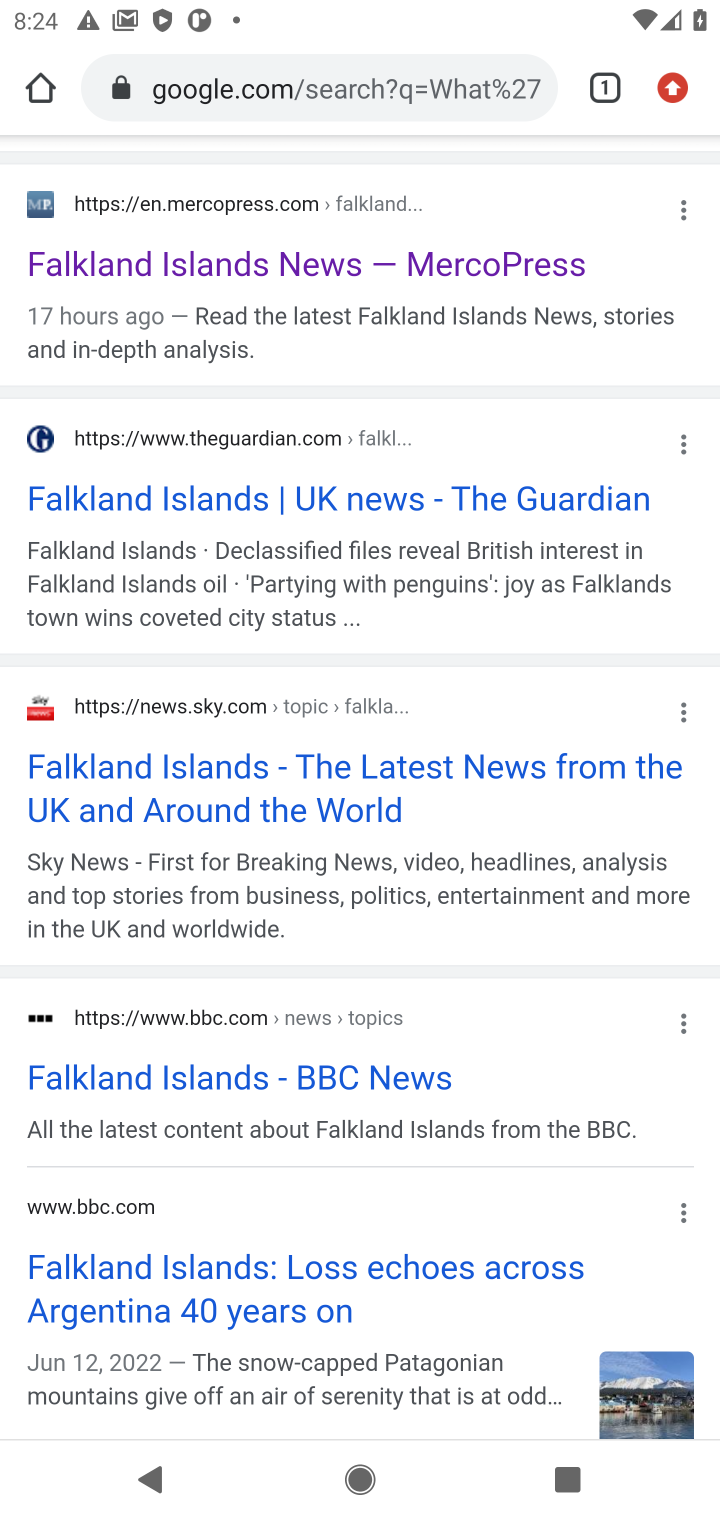
Step 29: click (232, 809)
Your task to perform on an android device: What's the news in theFalkland Islands? Image 30: 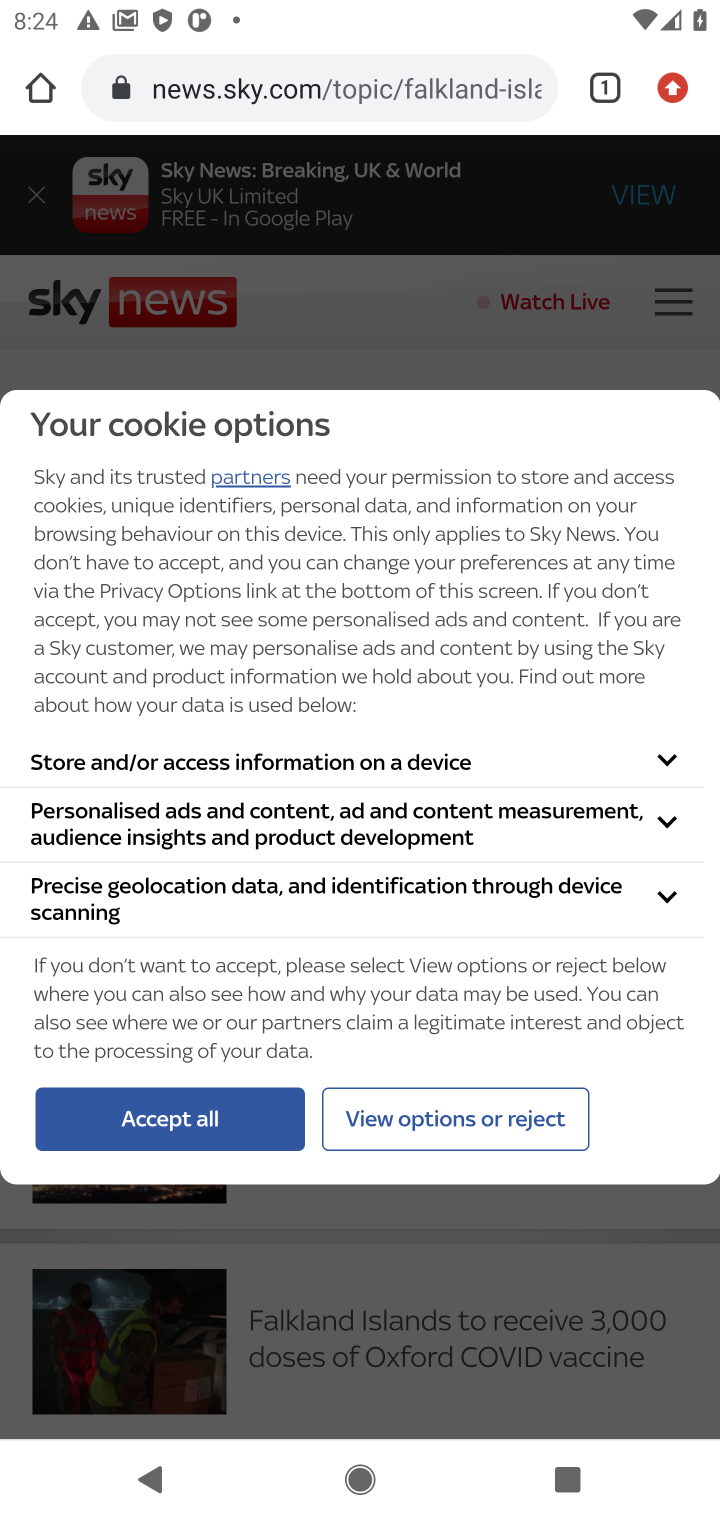
Step 30: click (208, 1125)
Your task to perform on an android device: What's the news in theFalkland Islands? Image 31: 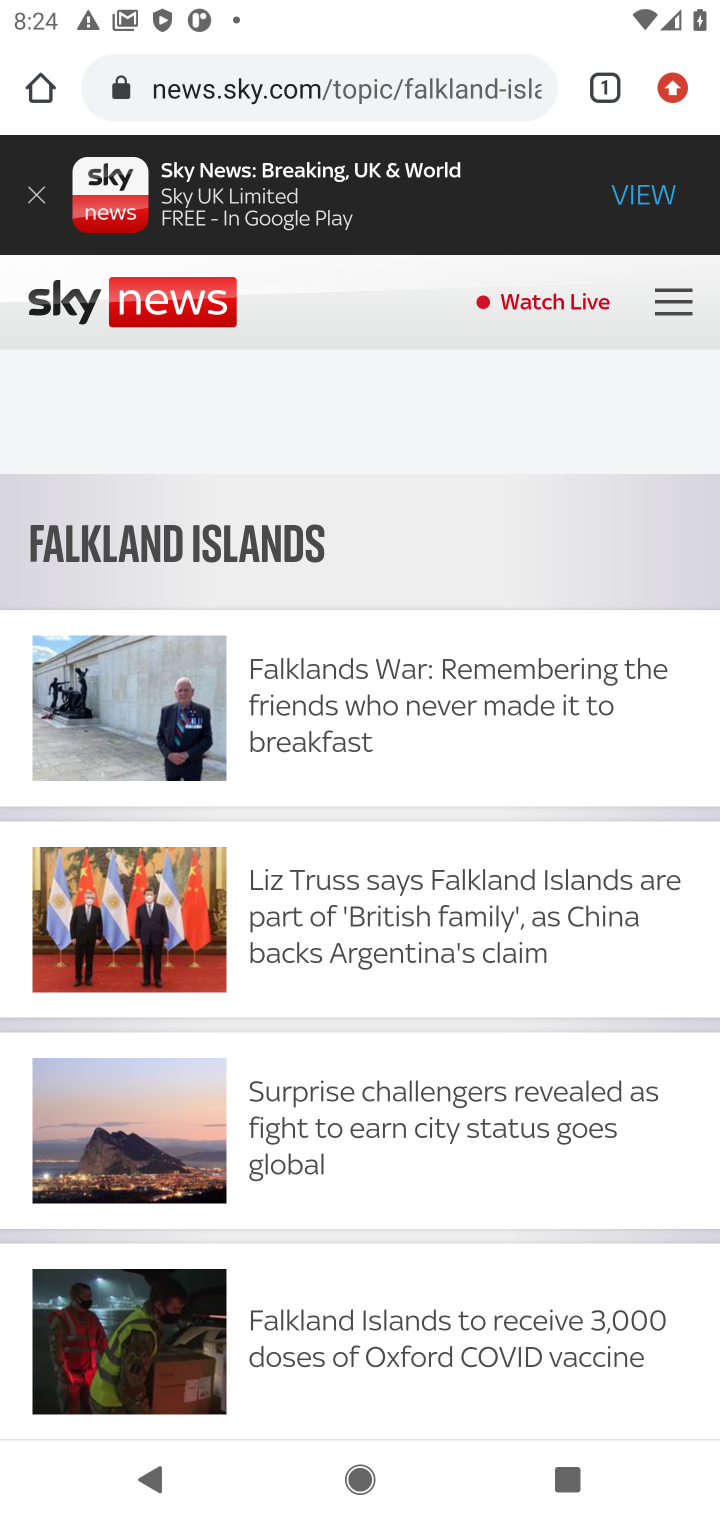
Step 31: drag from (302, 1196) to (373, 414)
Your task to perform on an android device: What's the news in theFalkland Islands? Image 32: 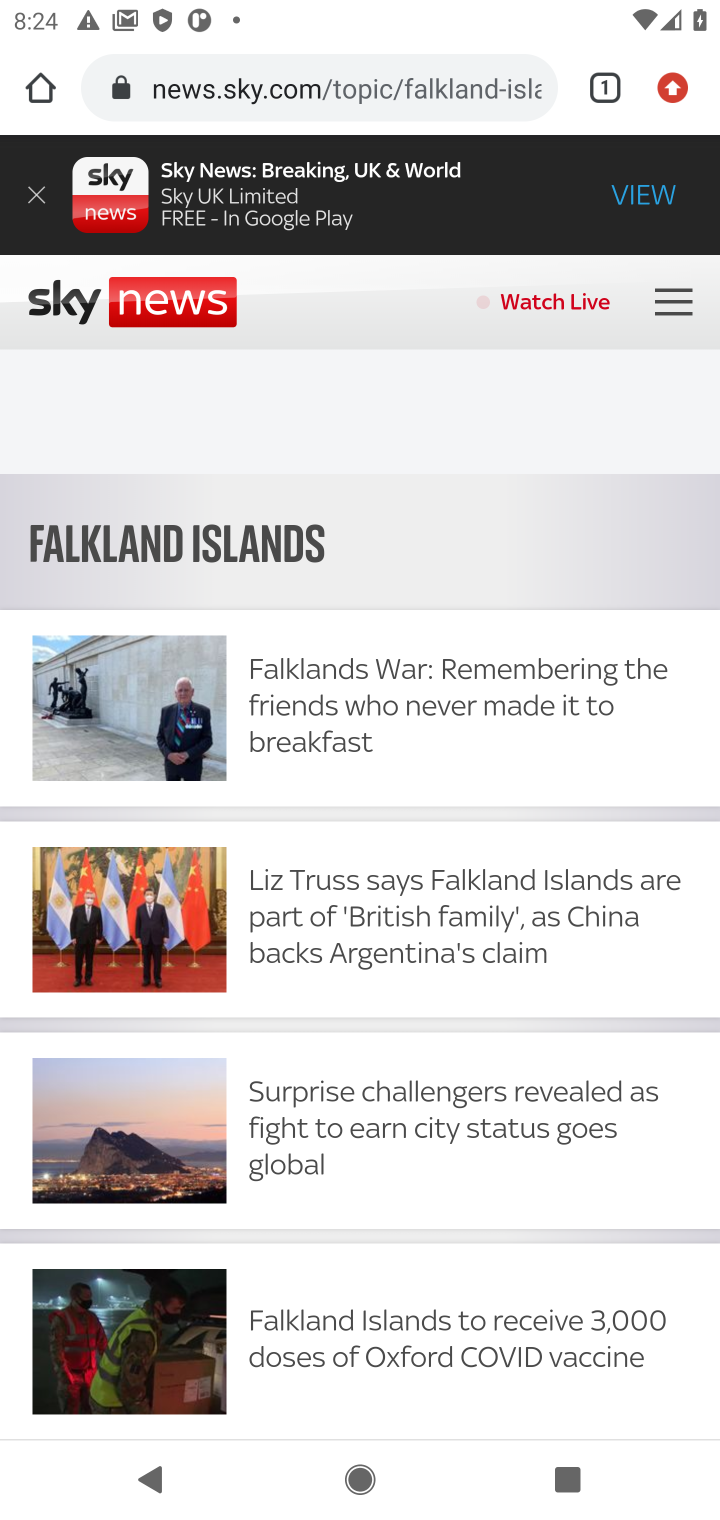
Step 32: drag from (377, 502) to (428, 363)
Your task to perform on an android device: What's the news in theFalkland Islands? Image 33: 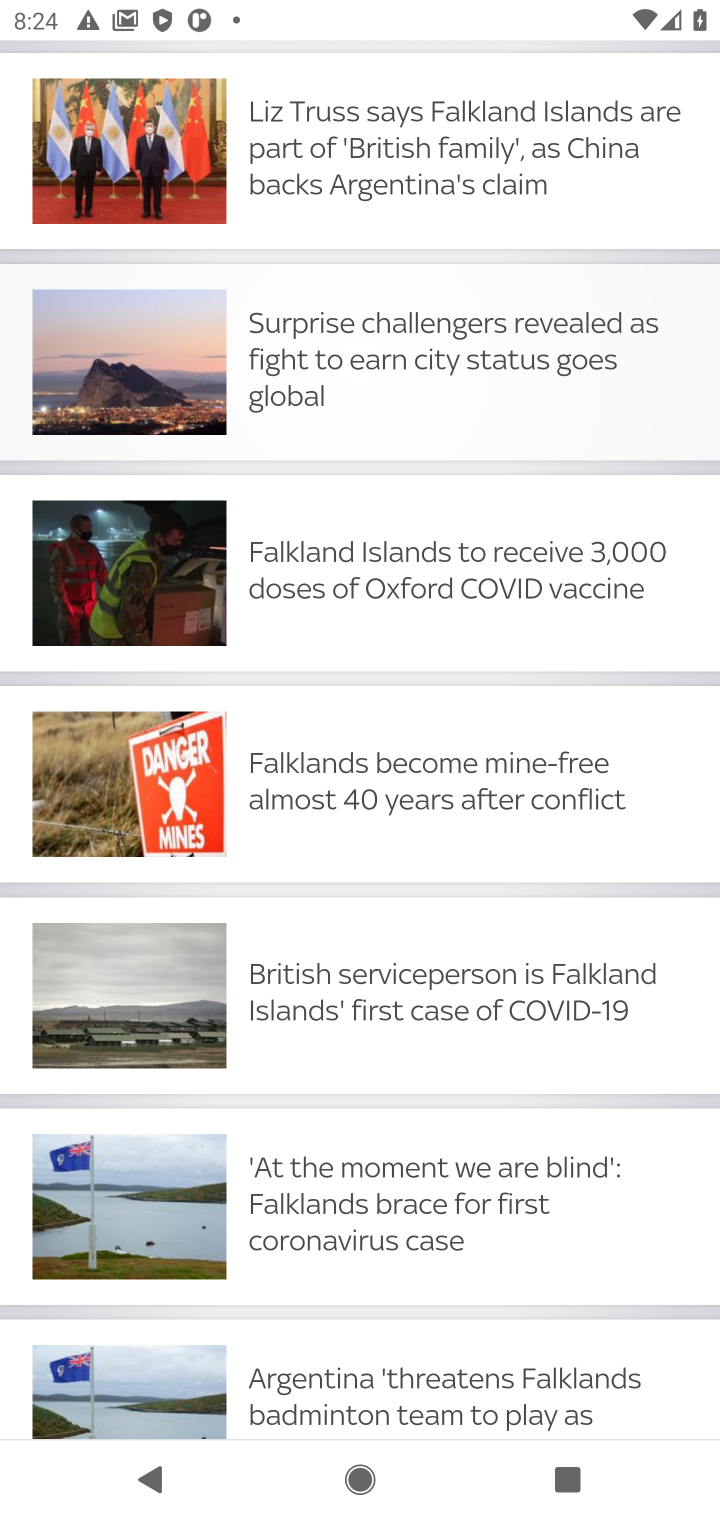
Step 33: drag from (390, 936) to (534, 313)
Your task to perform on an android device: What's the news in theFalkland Islands? Image 34: 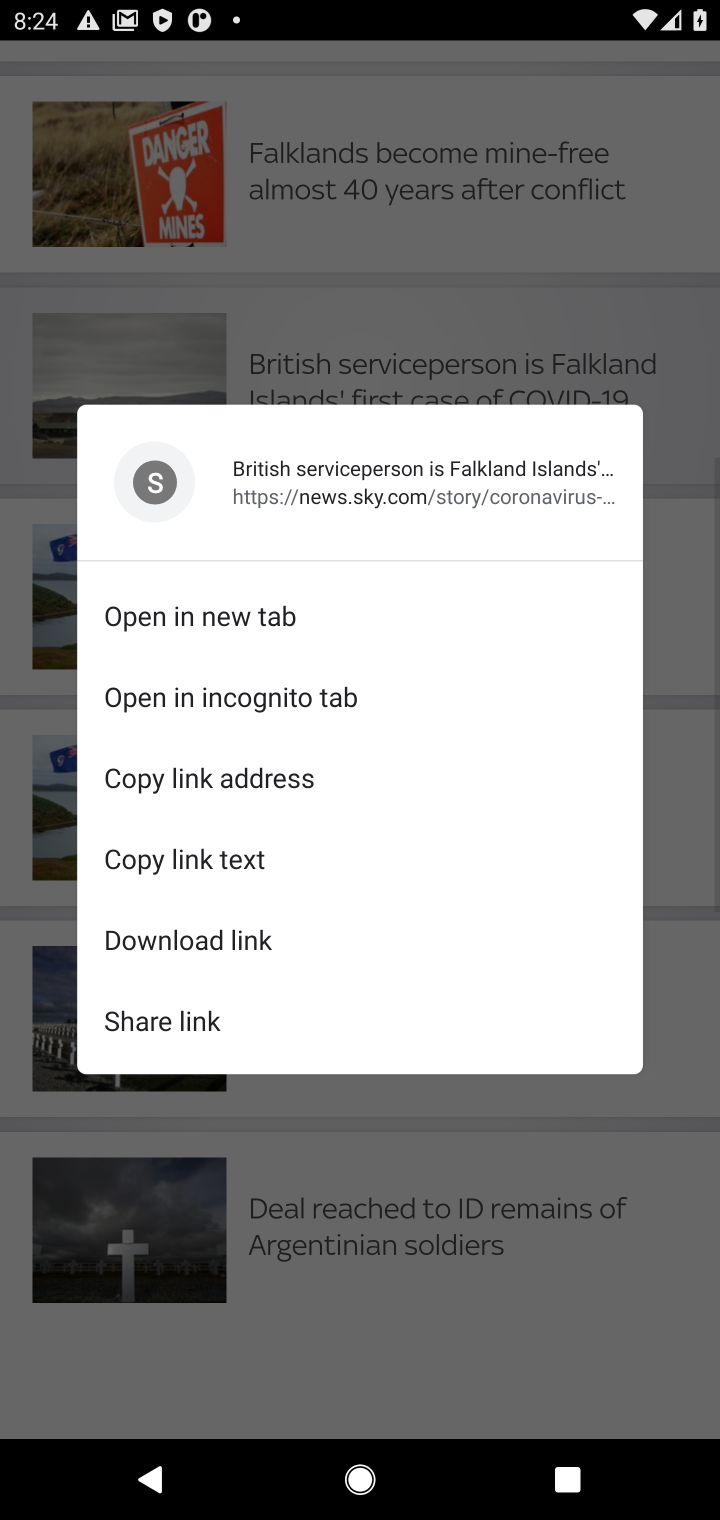
Step 34: drag from (408, 479) to (391, 298)
Your task to perform on an android device: What's the news in theFalkland Islands? Image 35: 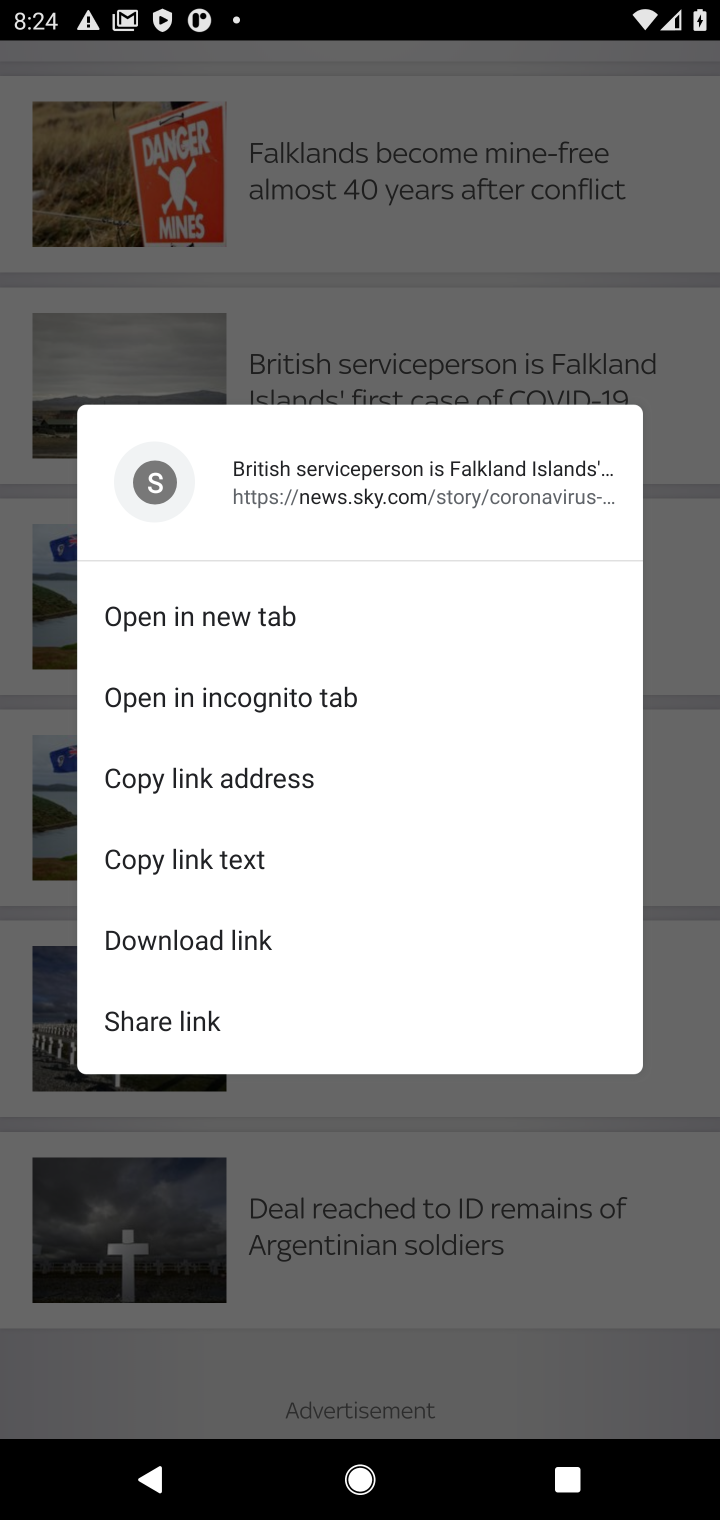
Step 35: click (391, 298)
Your task to perform on an android device: What's the news in theFalkland Islands? Image 36: 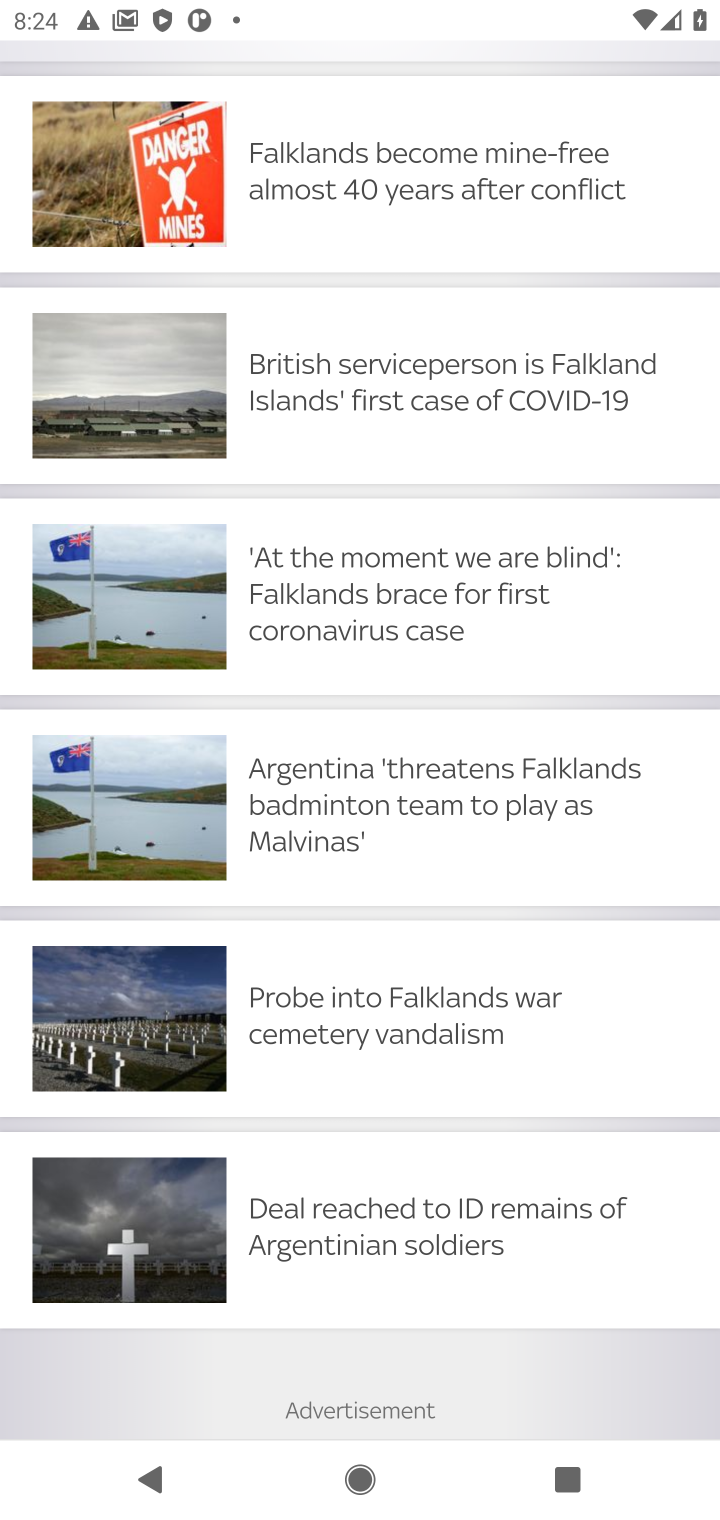
Step 36: drag from (425, 769) to (442, 222)
Your task to perform on an android device: What's the news in theFalkland Islands? Image 37: 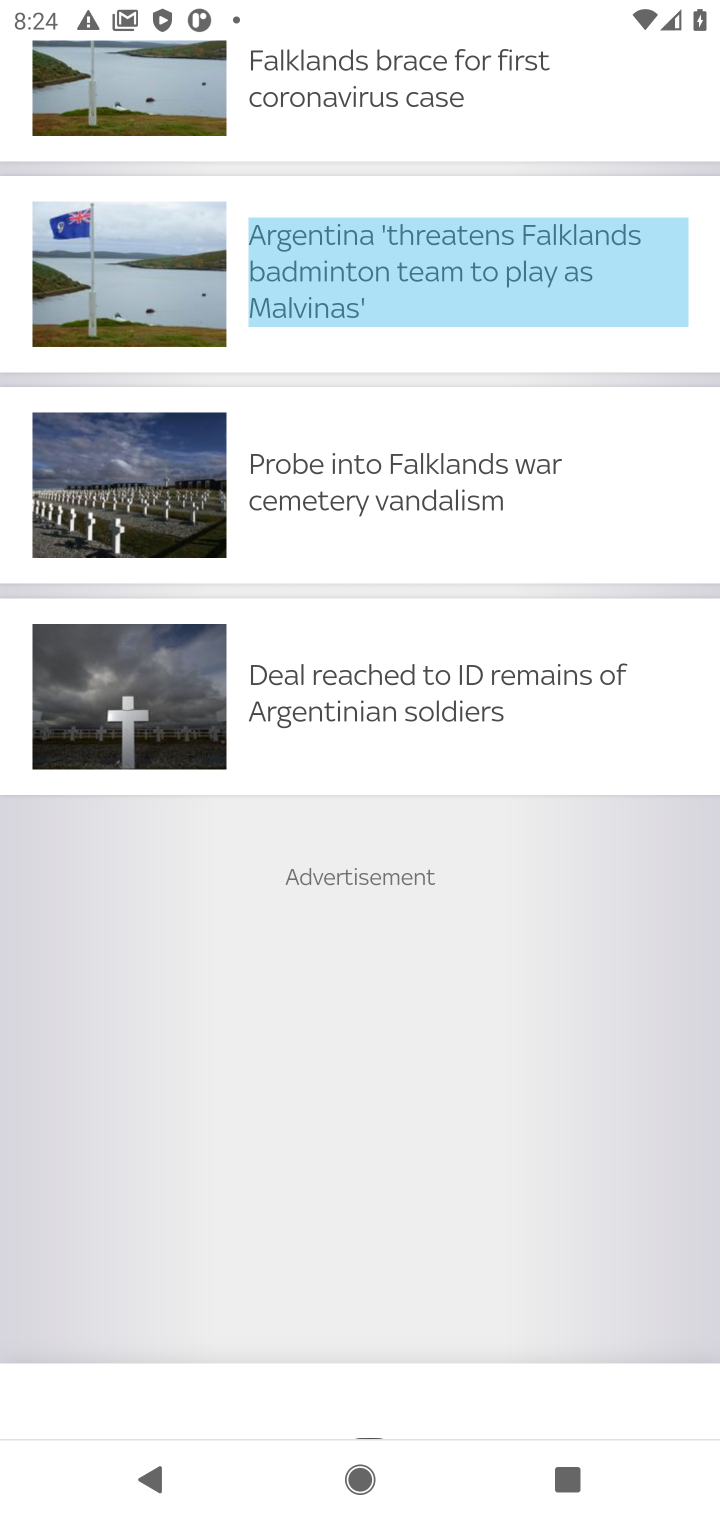
Step 37: drag from (383, 1116) to (401, 230)
Your task to perform on an android device: What's the news in theFalkland Islands? Image 38: 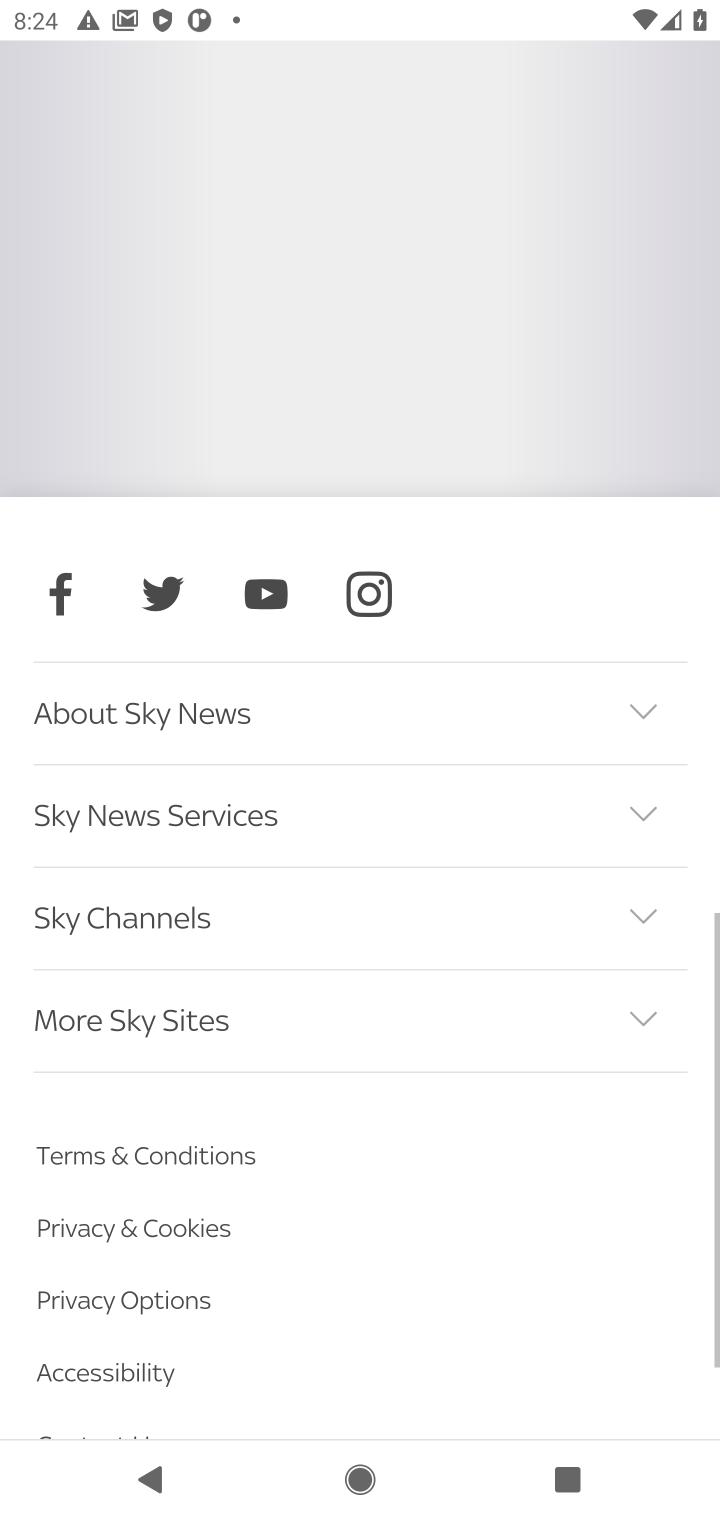
Step 38: drag from (364, 862) to (360, 1160)
Your task to perform on an android device: What's the news in theFalkland Islands? Image 39: 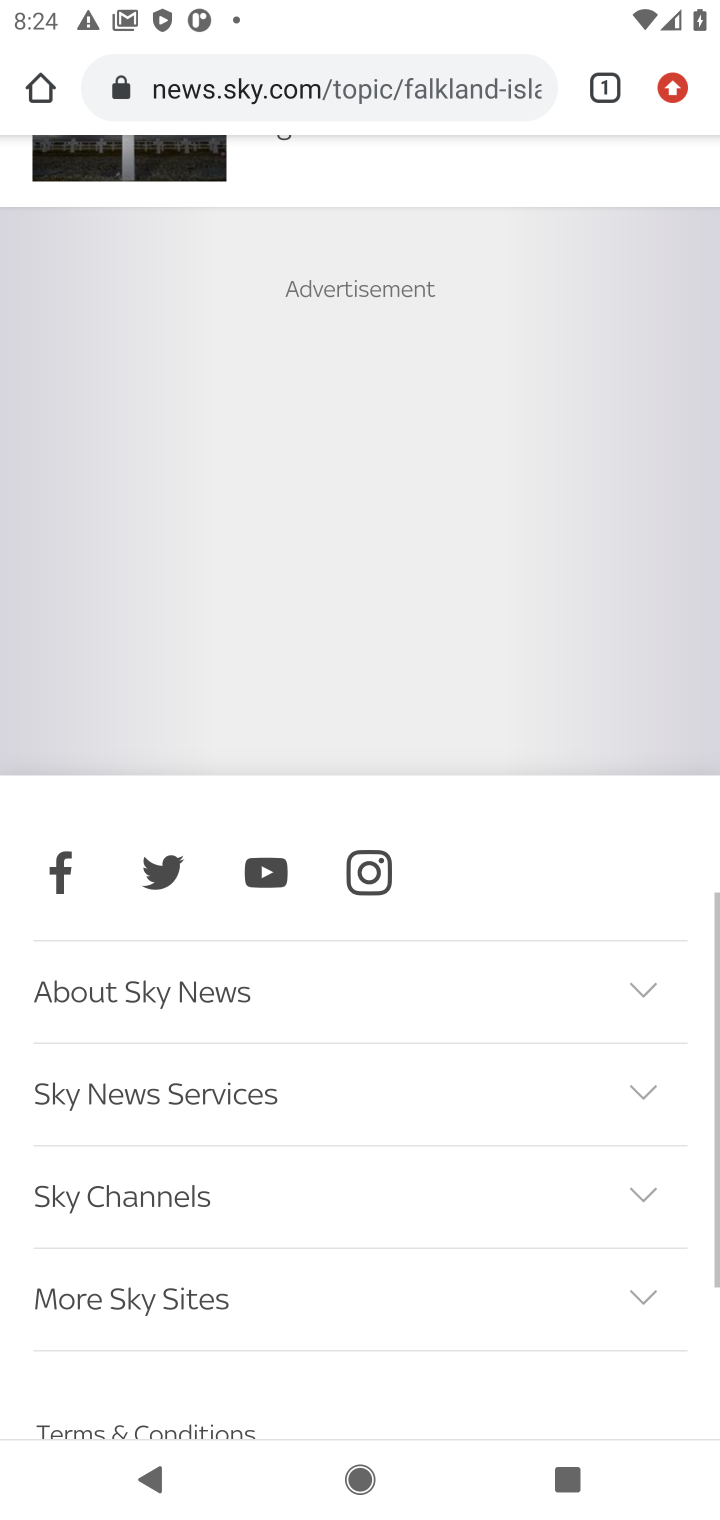
Step 39: drag from (365, 306) to (318, 938)
Your task to perform on an android device: What's the news in theFalkland Islands? Image 40: 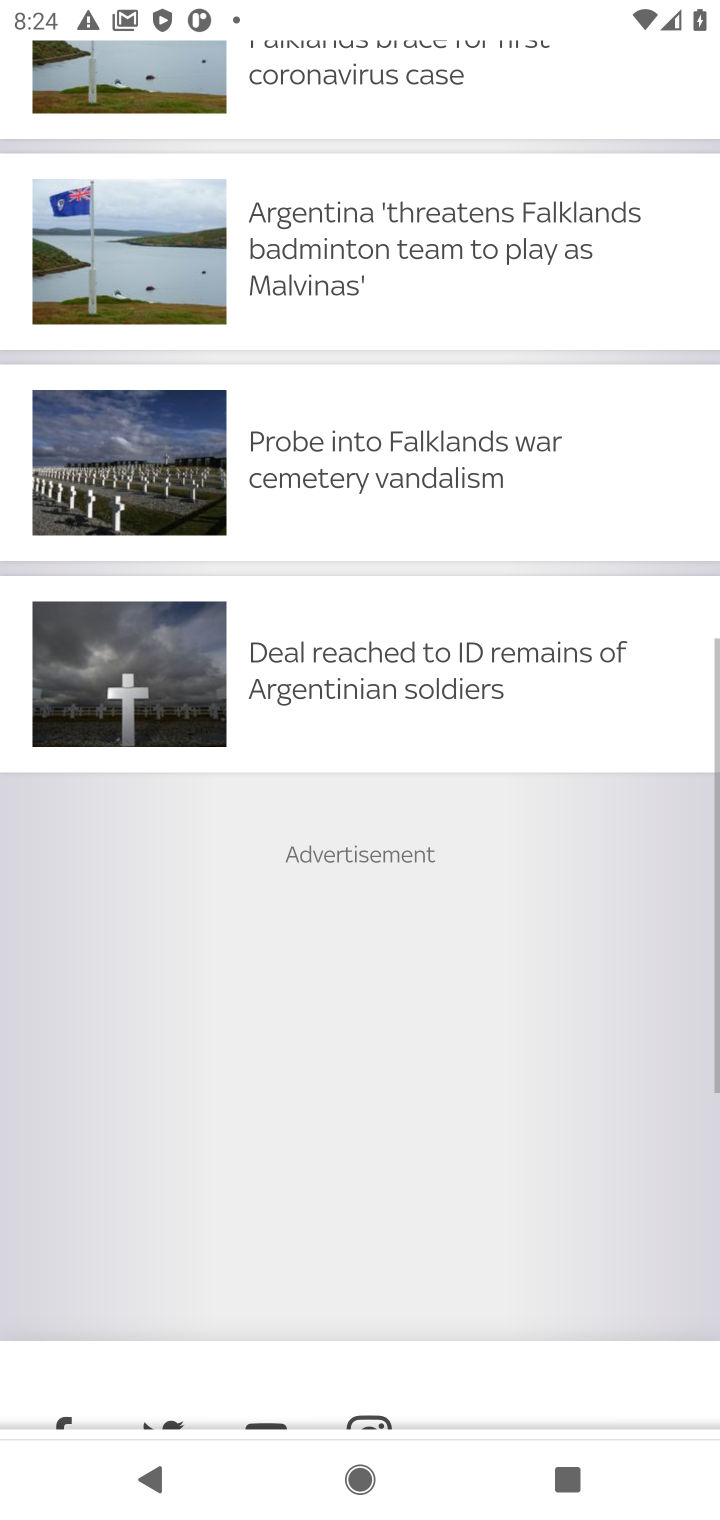
Step 40: drag from (372, 696) to (373, 987)
Your task to perform on an android device: What's the news in theFalkland Islands? Image 41: 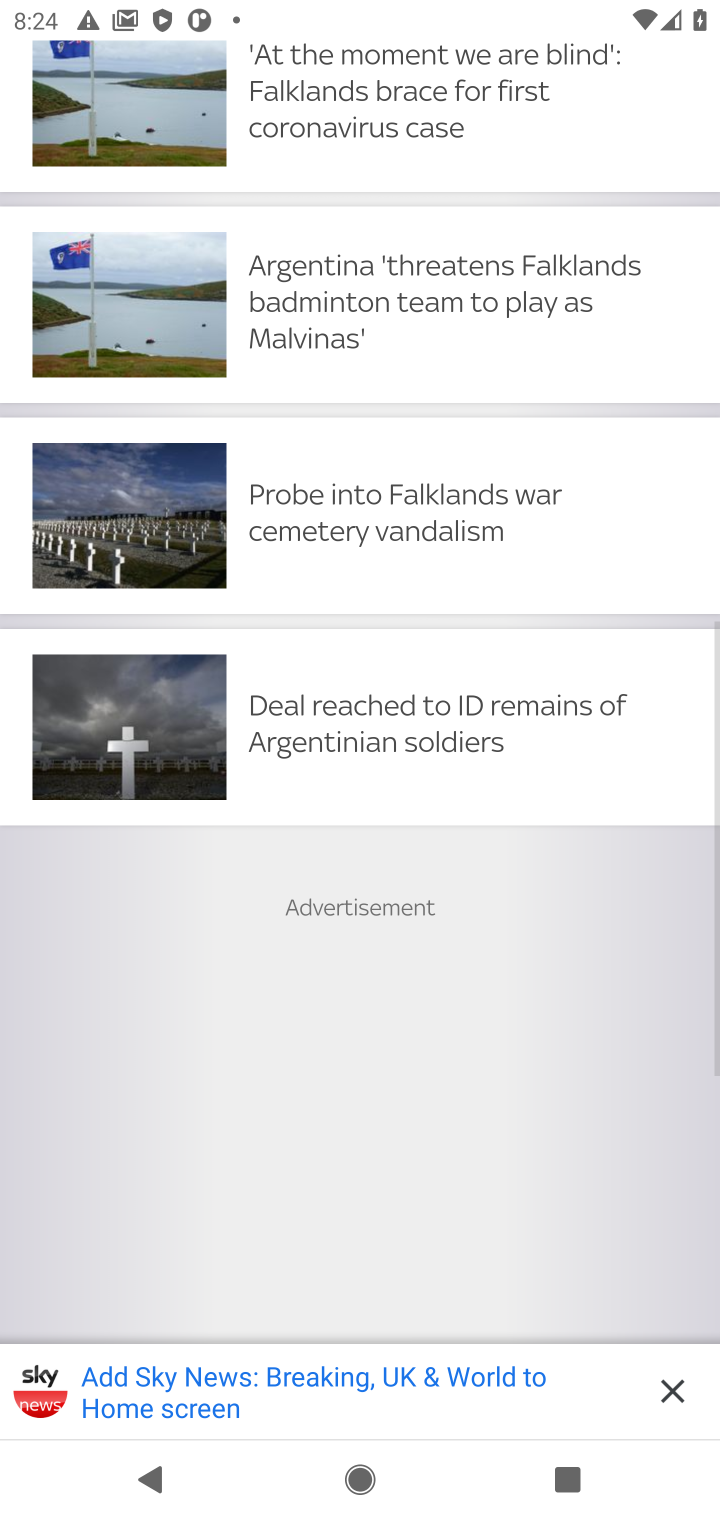
Step 41: drag from (375, 474) to (385, 933)
Your task to perform on an android device: What's the news in theFalkland Islands? Image 42: 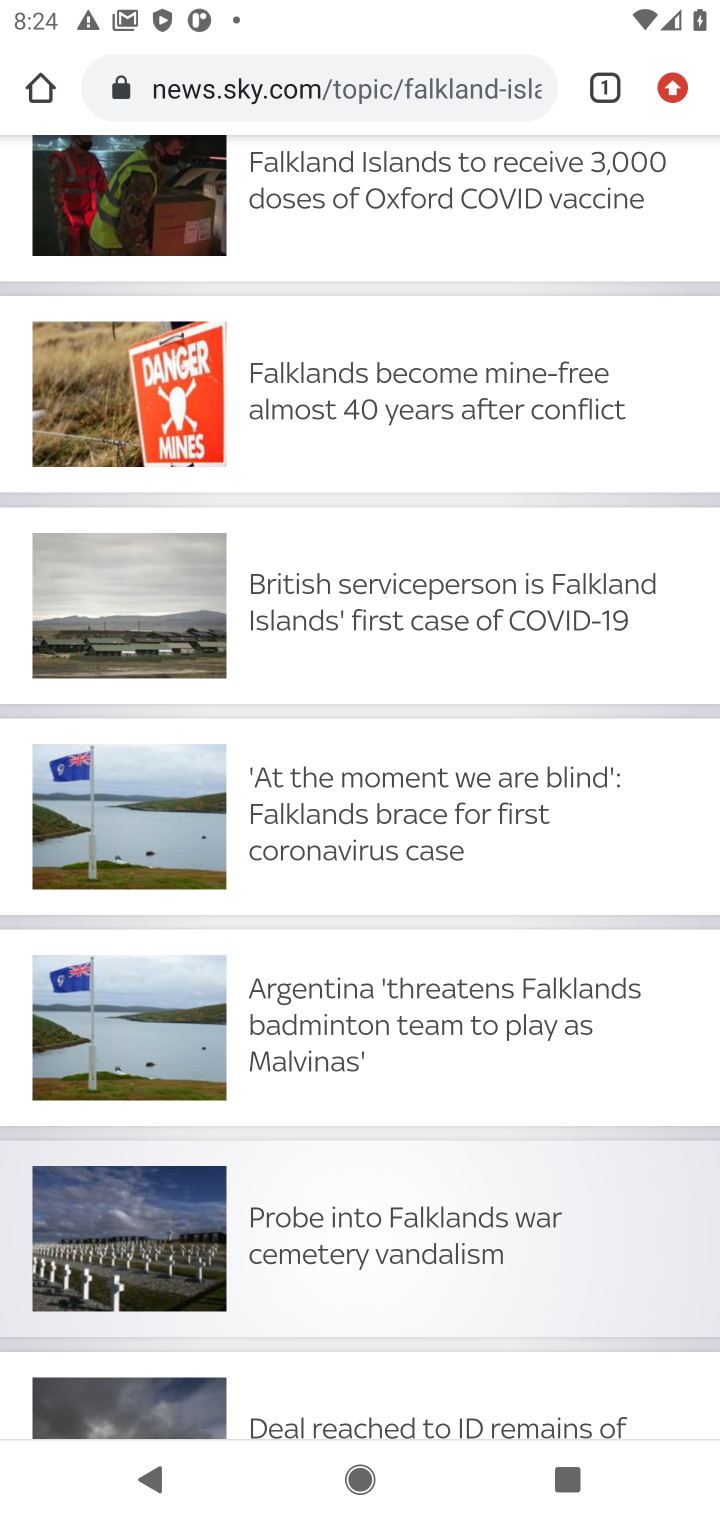
Step 42: drag from (365, 839) to (390, 1051)
Your task to perform on an android device: What's the news in theFalkland Islands? Image 43: 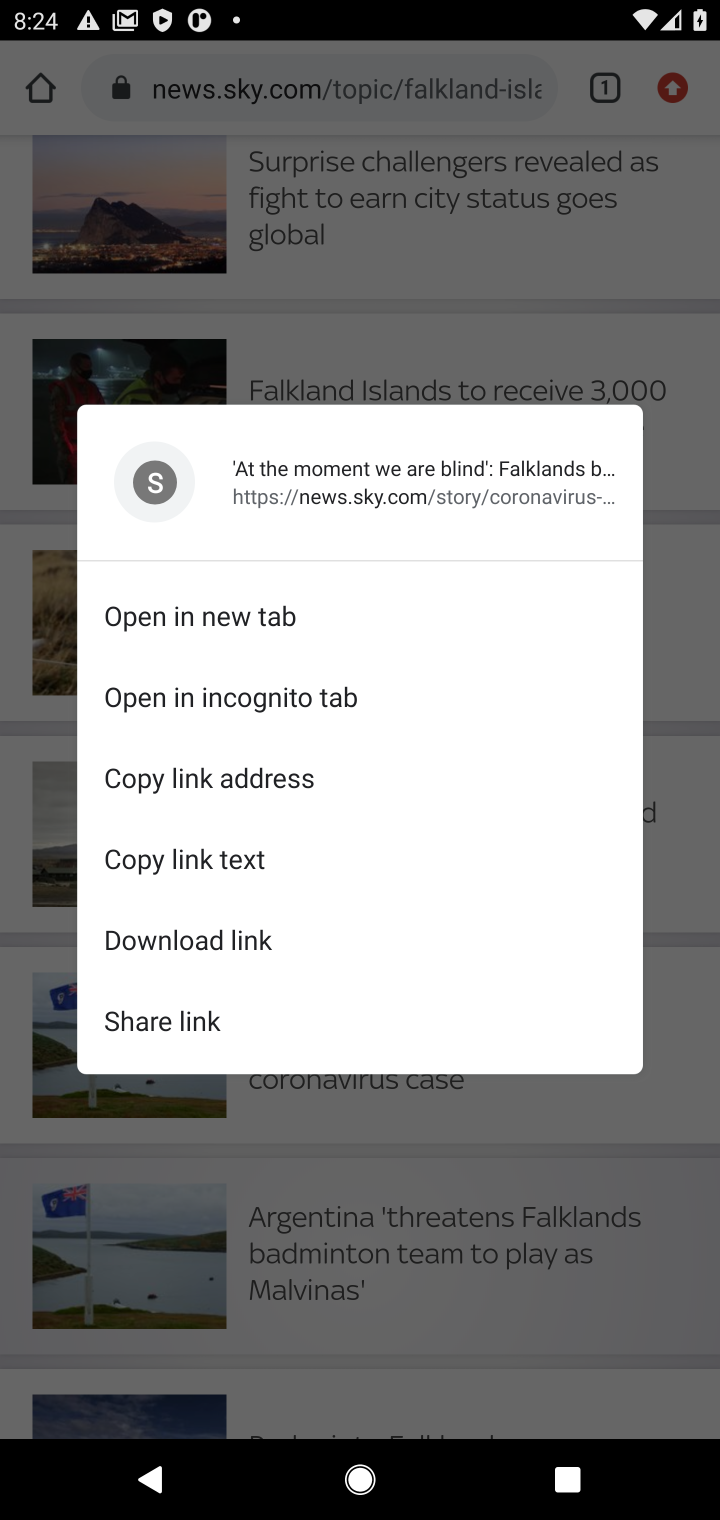
Step 43: click (449, 340)
Your task to perform on an android device: What's the news in theFalkland Islands? Image 44: 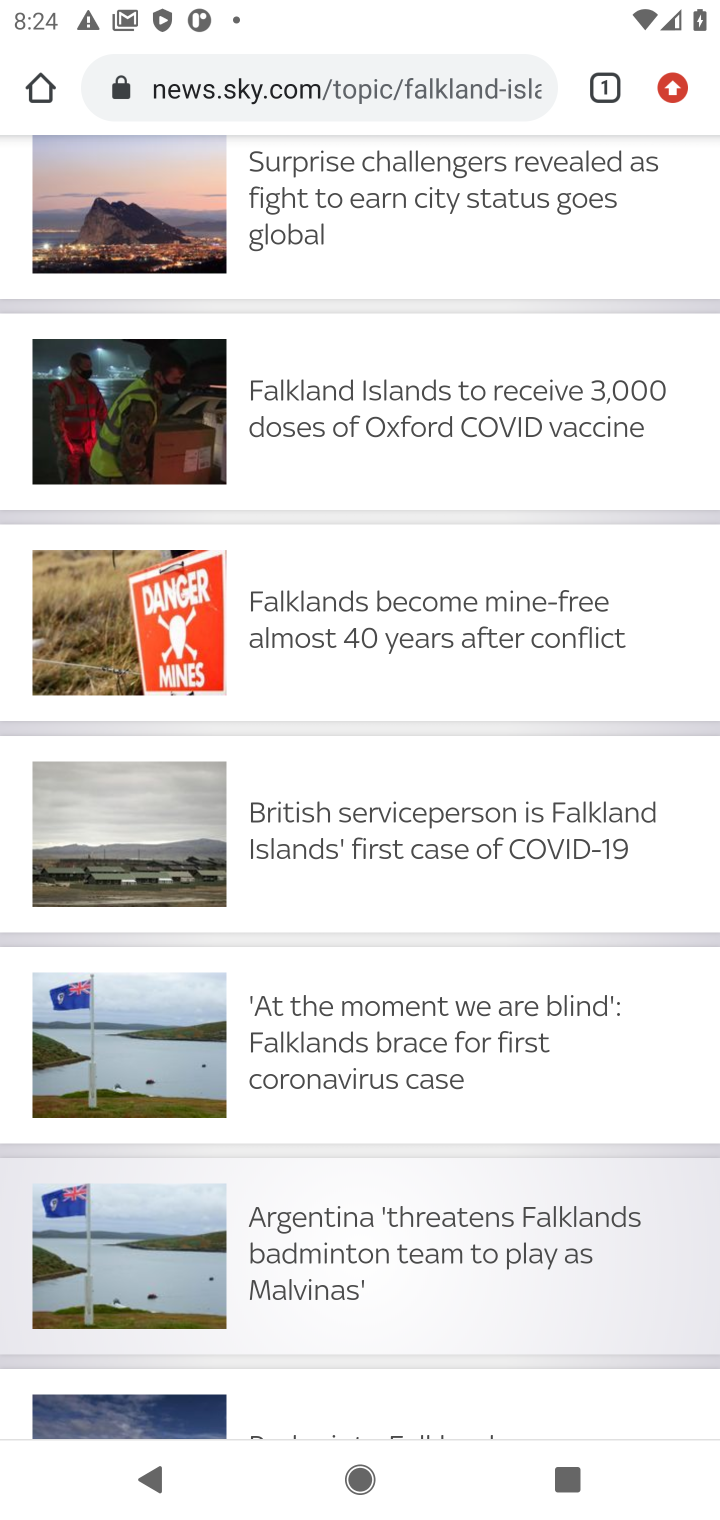
Step 44: press back button
Your task to perform on an android device: What's the news in theFalkland Islands? Image 45: 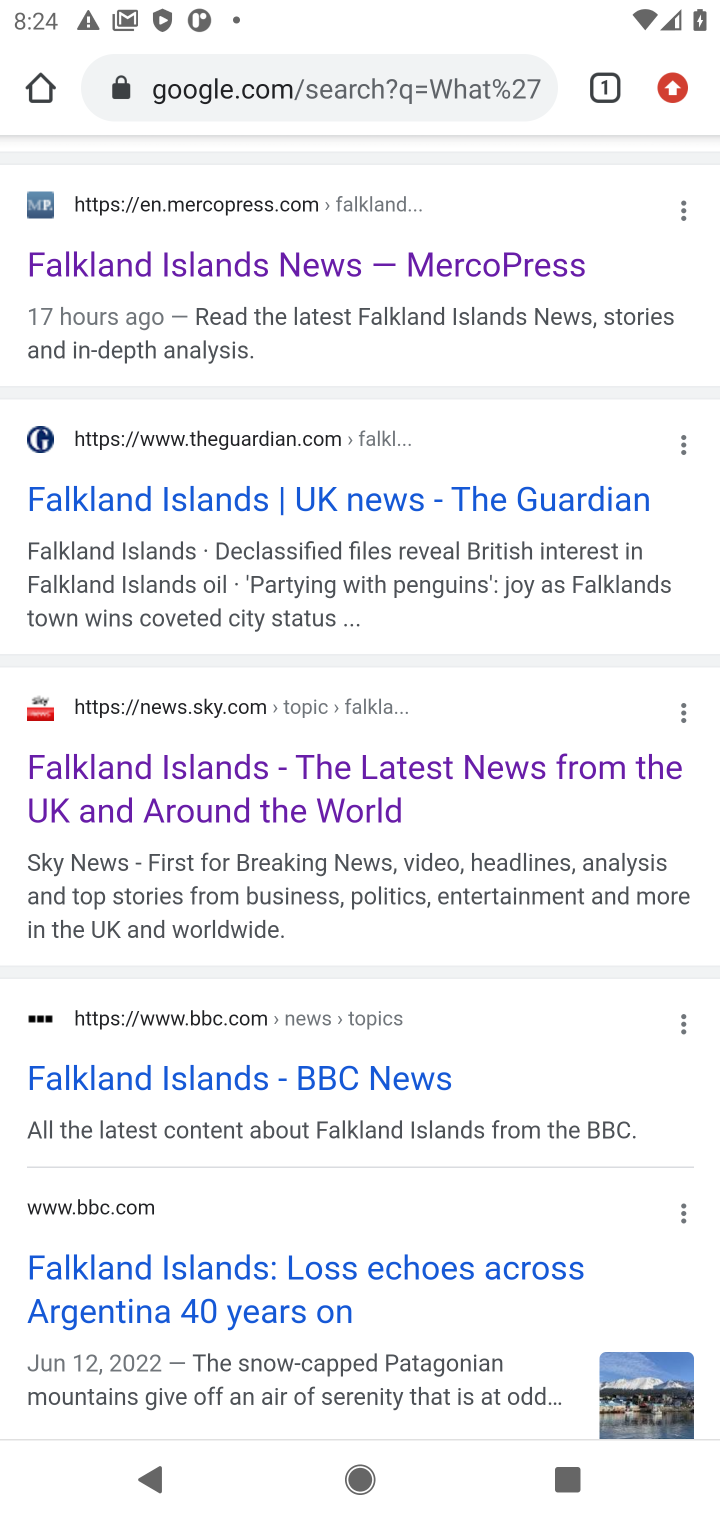
Step 45: click (322, 504)
Your task to perform on an android device: What's the news in theFalkland Islands? Image 46: 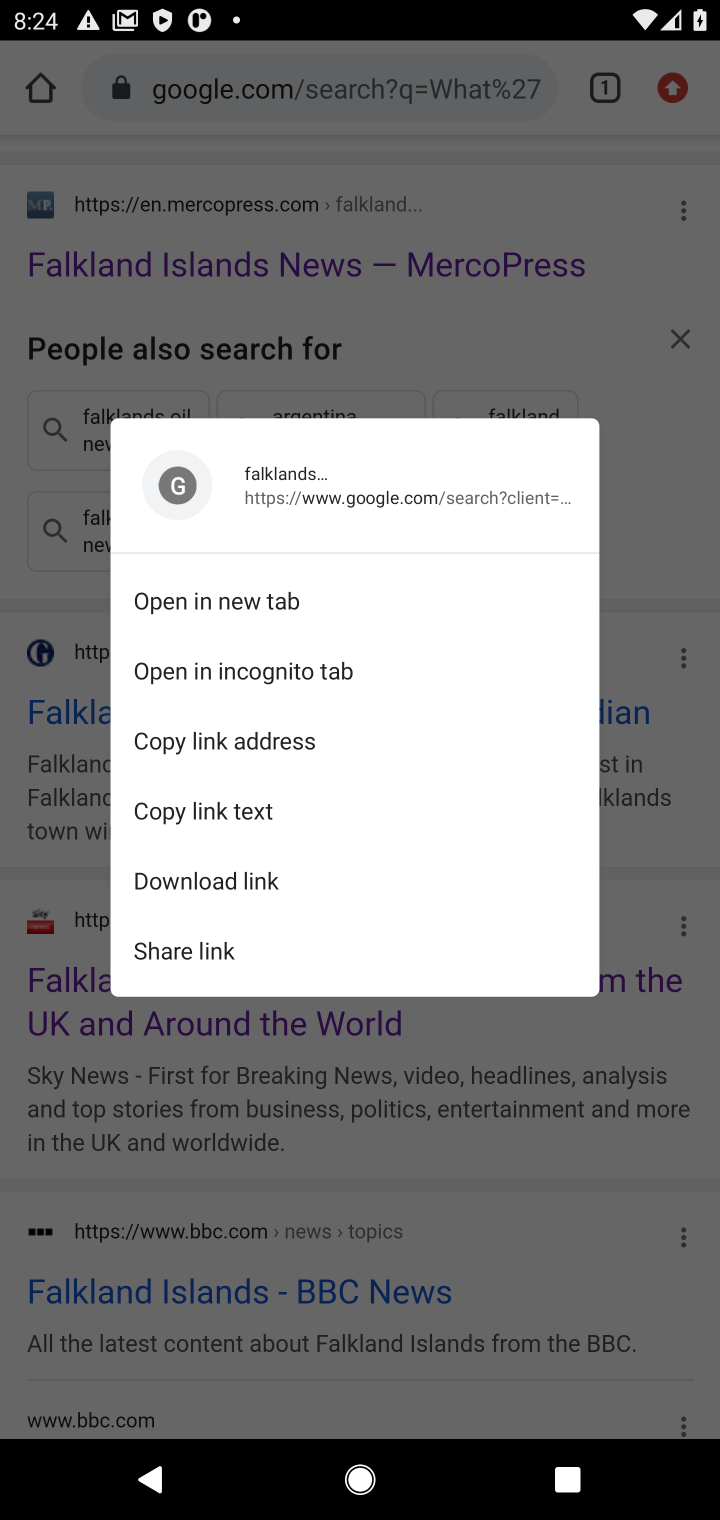
Step 46: click (221, 719)
Your task to perform on an android device: What's the news in theFalkland Islands? Image 47: 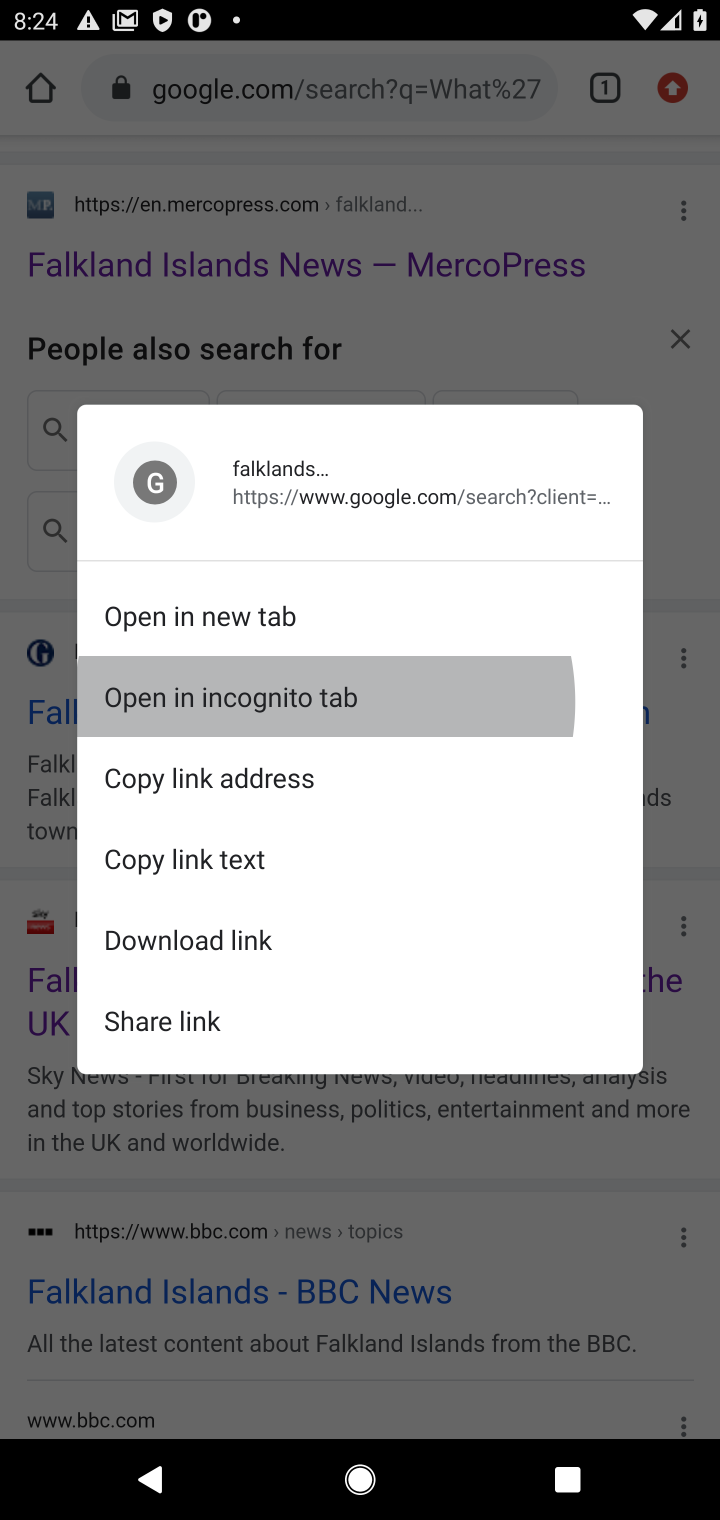
Step 47: click (384, 325)
Your task to perform on an android device: What's the news in theFalkland Islands? Image 48: 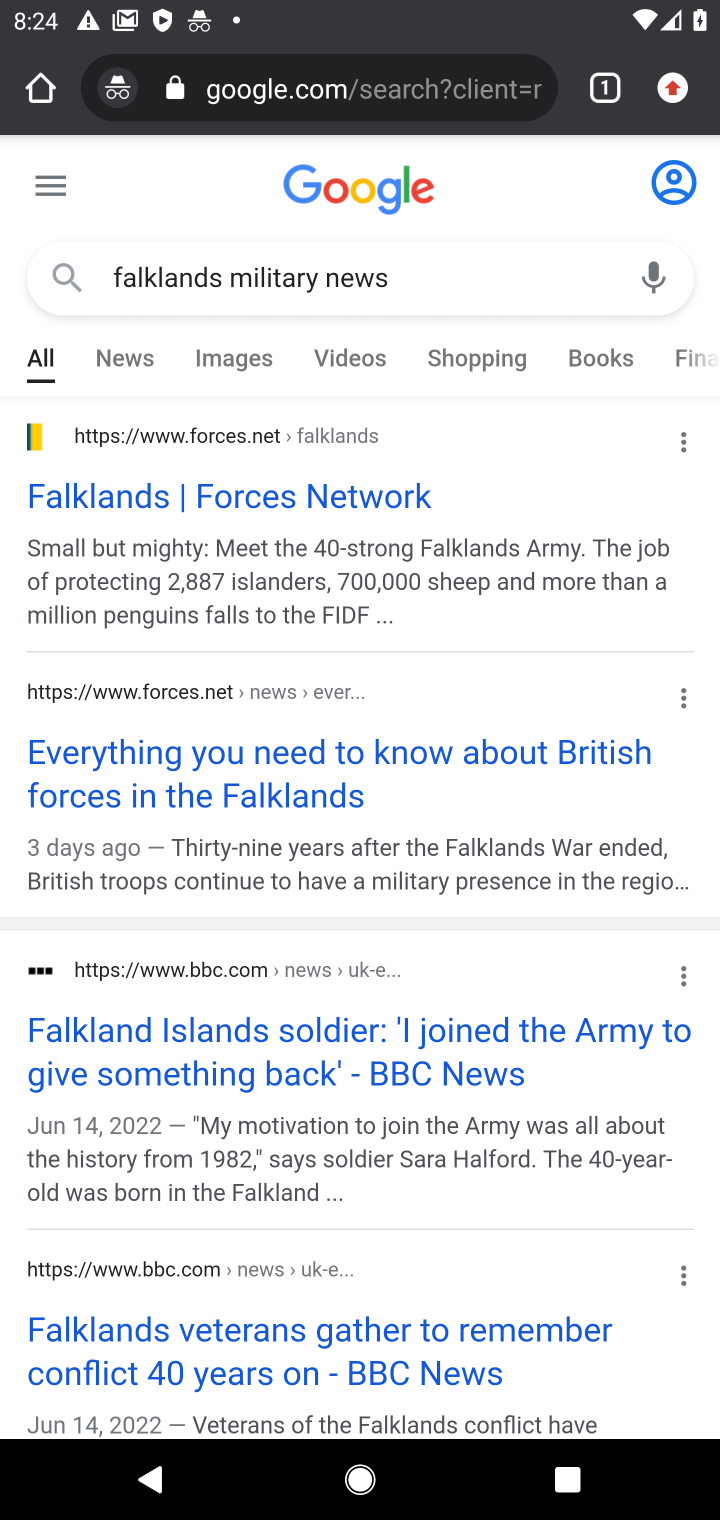
Step 48: click (247, 1043)
Your task to perform on an android device: What's the news in theFalkland Islands? Image 49: 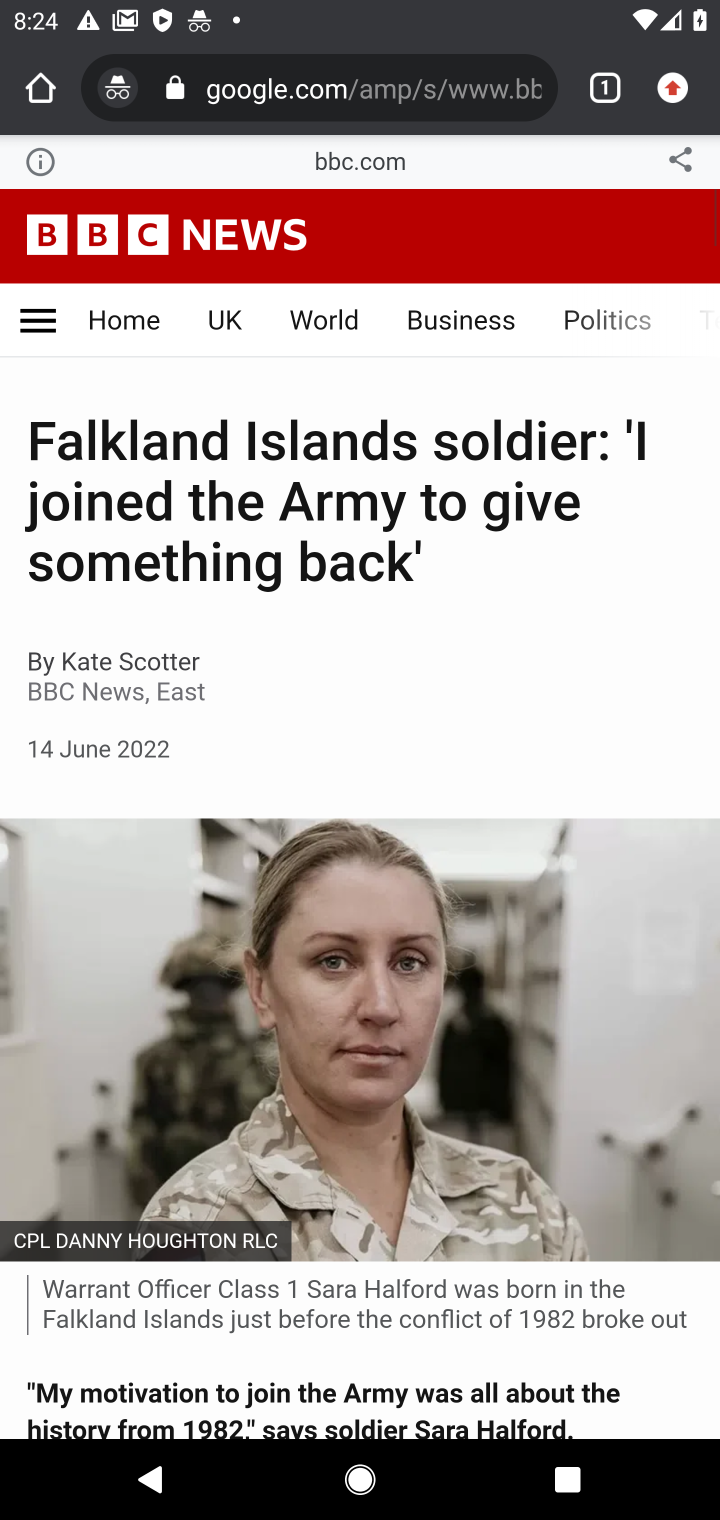
Step 49: drag from (331, 825) to (446, 358)
Your task to perform on an android device: What's the news in theFalkland Islands? Image 50: 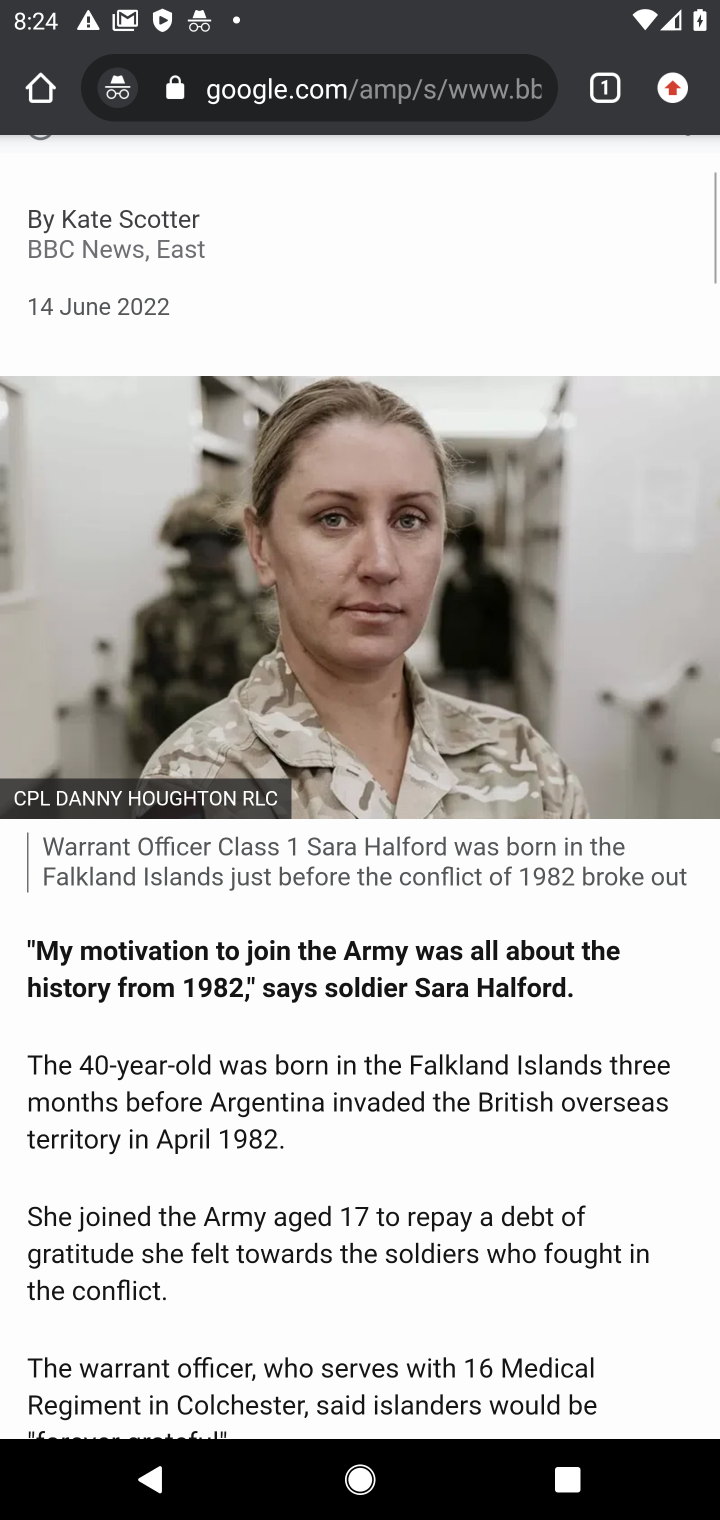
Step 50: drag from (458, 1175) to (487, 454)
Your task to perform on an android device: What's the news in theFalkland Islands? Image 51: 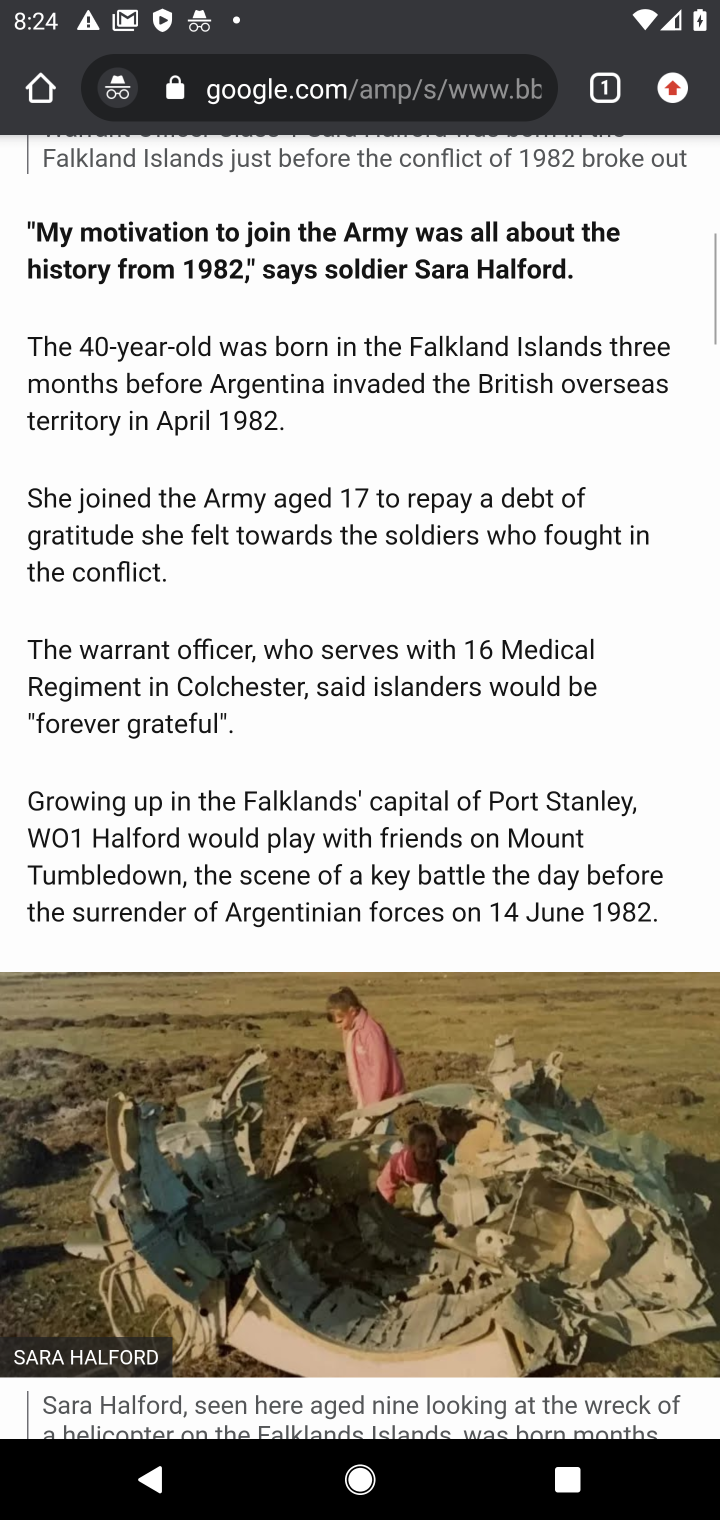
Step 51: drag from (276, 1339) to (322, 442)
Your task to perform on an android device: What's the news in theFalkland Islands? Image 52: 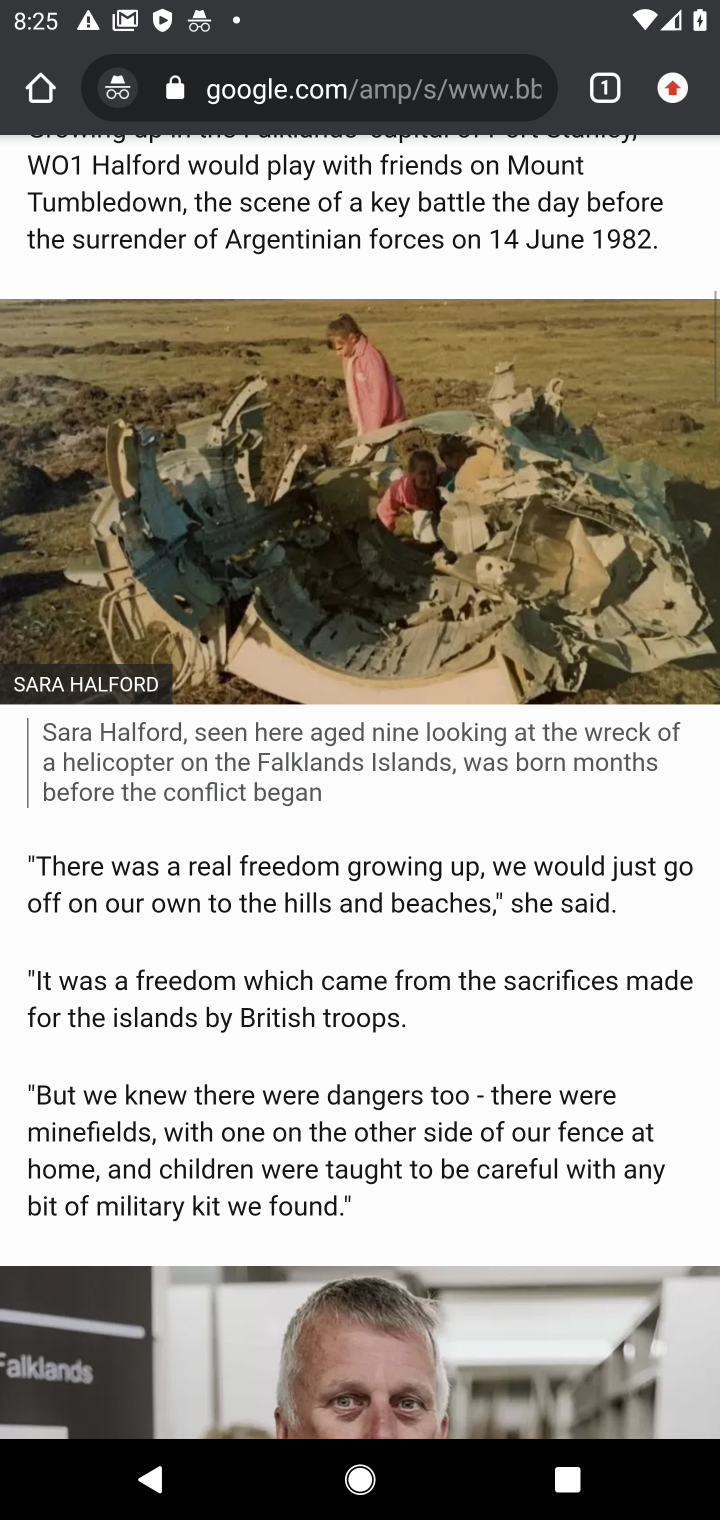
Step 52: click (362, 453)
Your task to perform on an android device: What's the news in theFalkland Islands? Image 53: 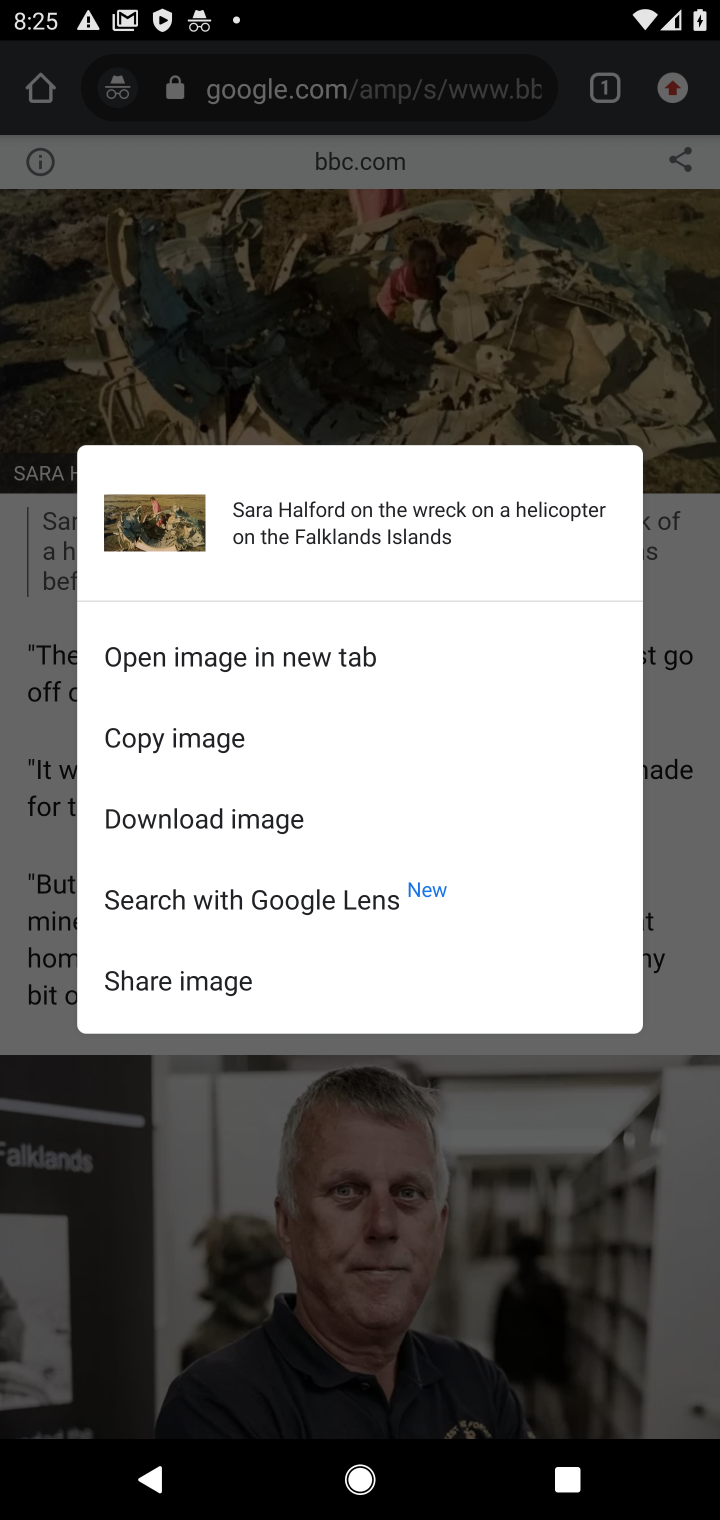
Step 53: click (366, 1273)
Your task to perform on an android device: What's the news in theFalkland Islands? Image 54: 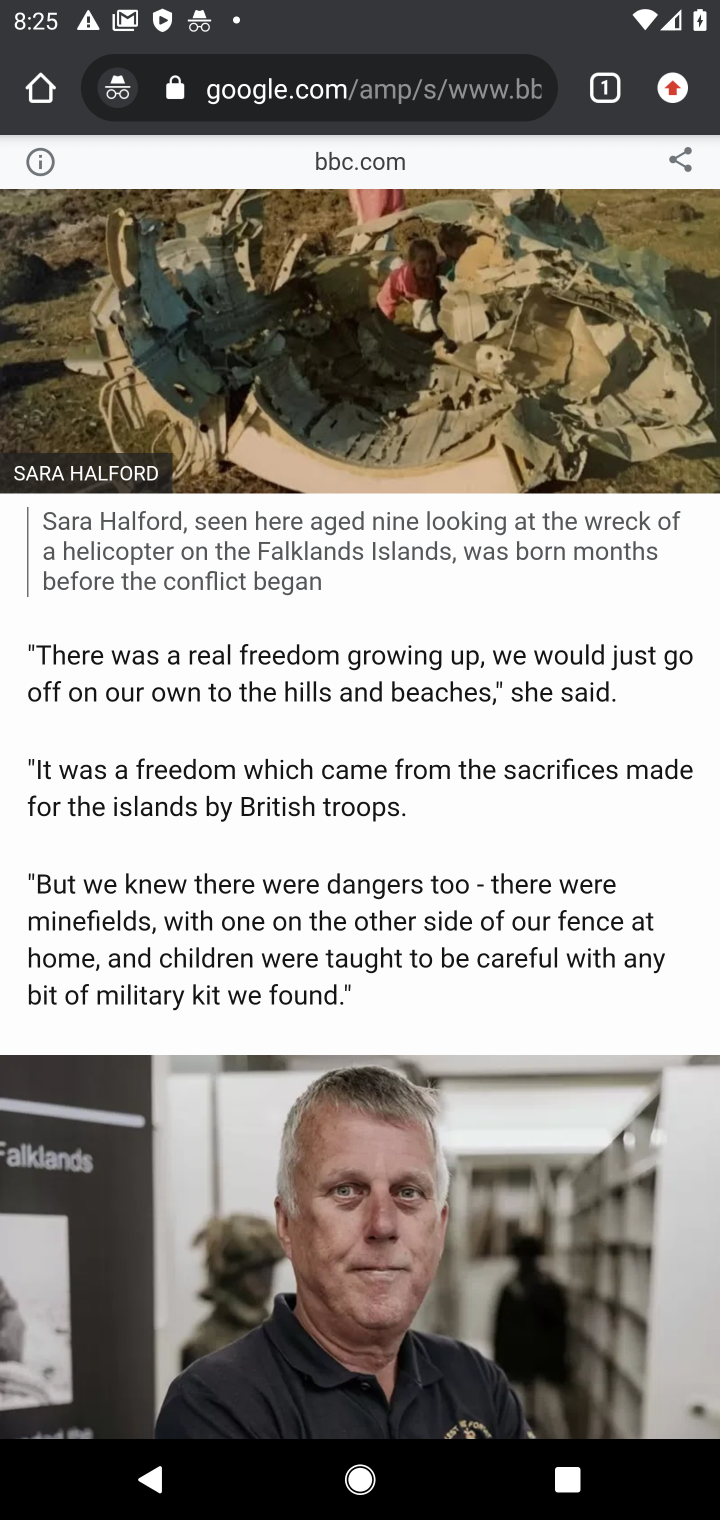
Step 54: drag from (549, 811) to (513, 359)
Your task to perform on an android device: What's the news in theFalkland Islands? Image 55: 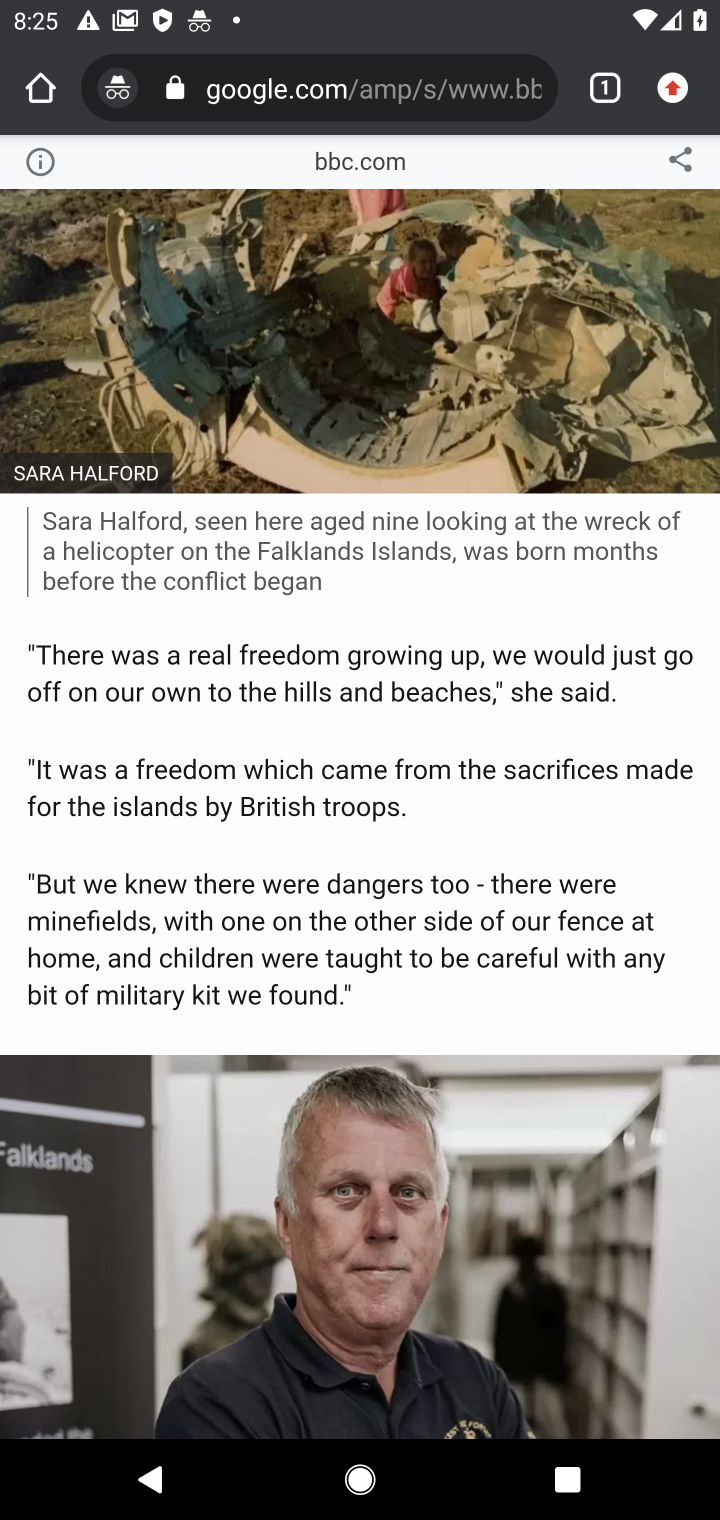
Step 55: click (387, 408)
Your task to perform on an android device: What's the news in theFalkland Islands? Image 56: 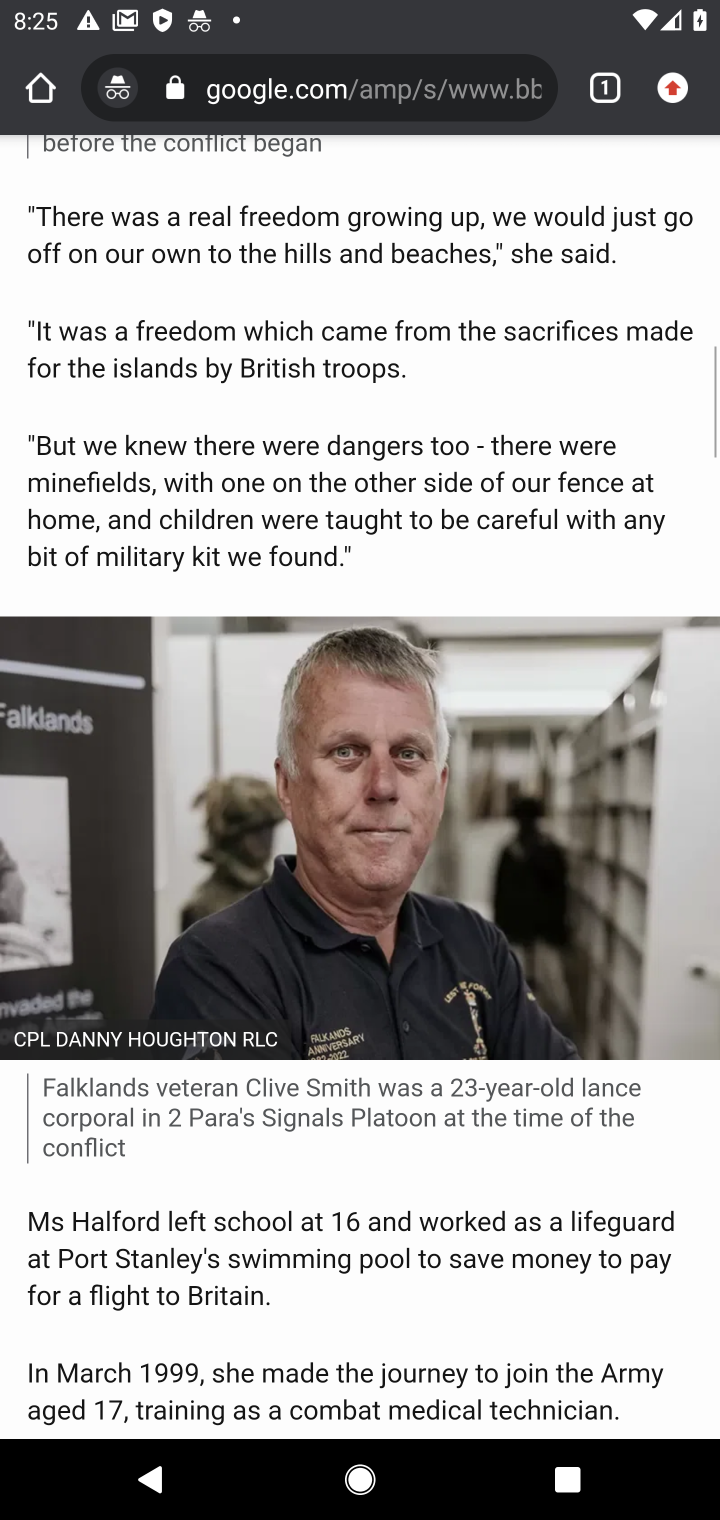
Step 56: drag from (336, 892) to (406, 295)
Your task to perform on an android device: What's the news in theFalkland Islands? Image 57: 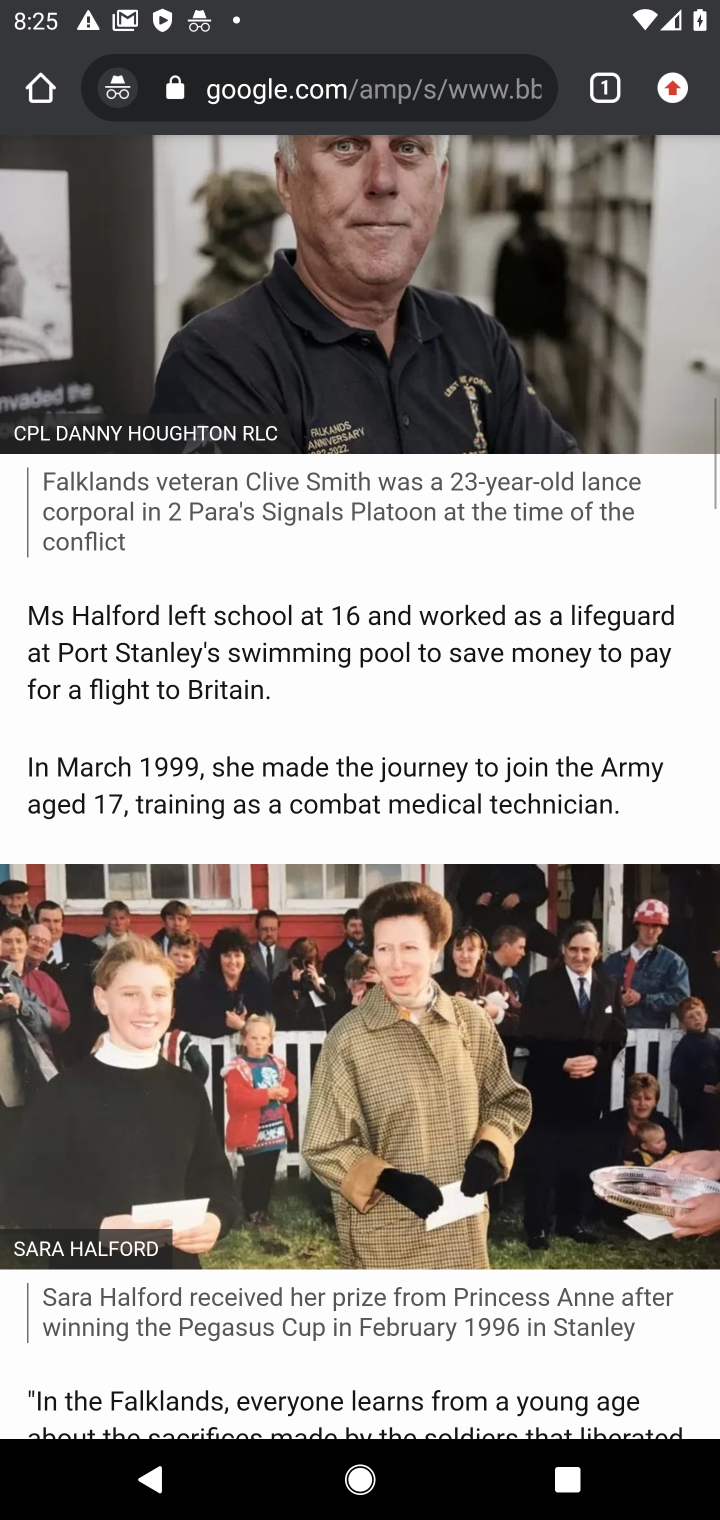
Step 57: drag from (584, 1102) to (649, 227)
Your task to perform on an android device: What's the news in theFalkland Islands? Image 58: 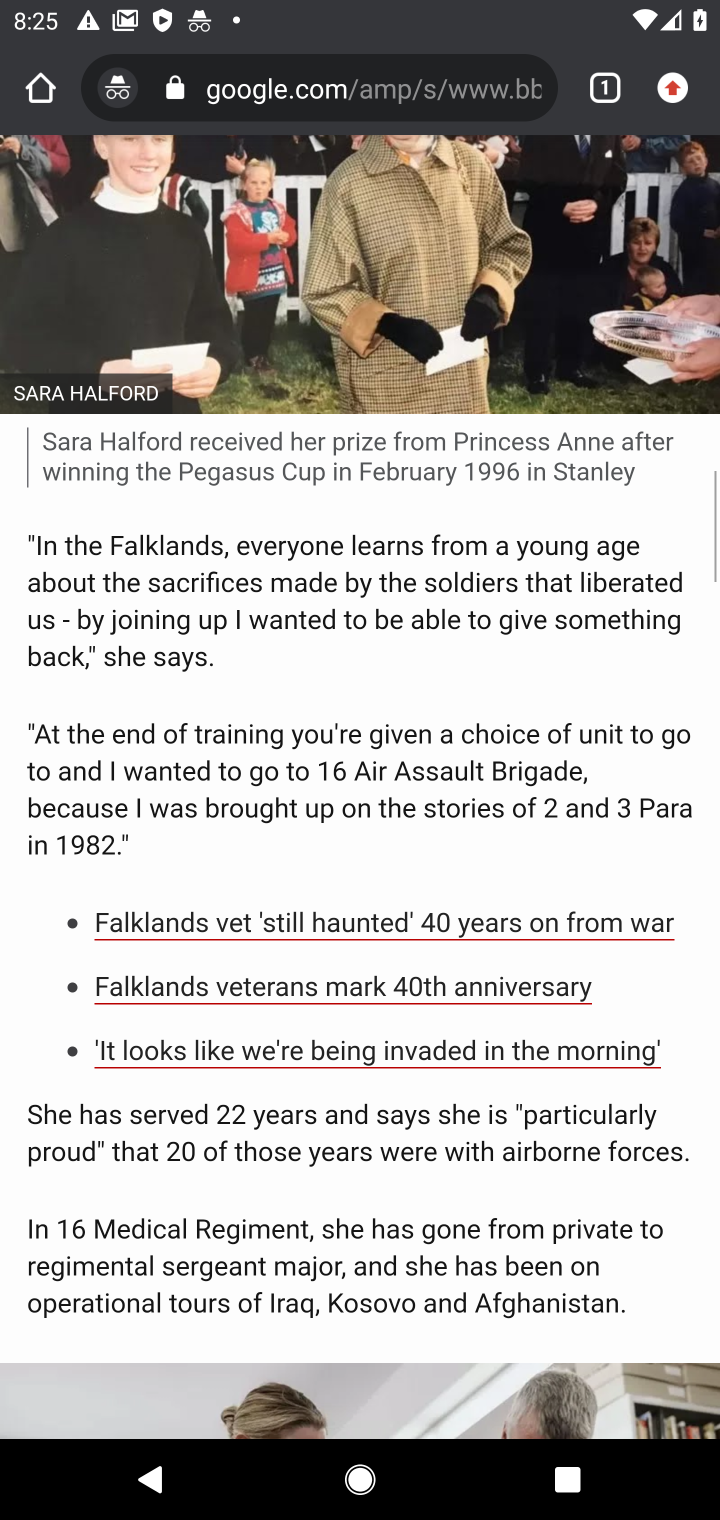
Step 58: drag from (420, 484) to (413, 238)
Your task to perform on an android device: What's the news in theFalkland Islands? Image 59: 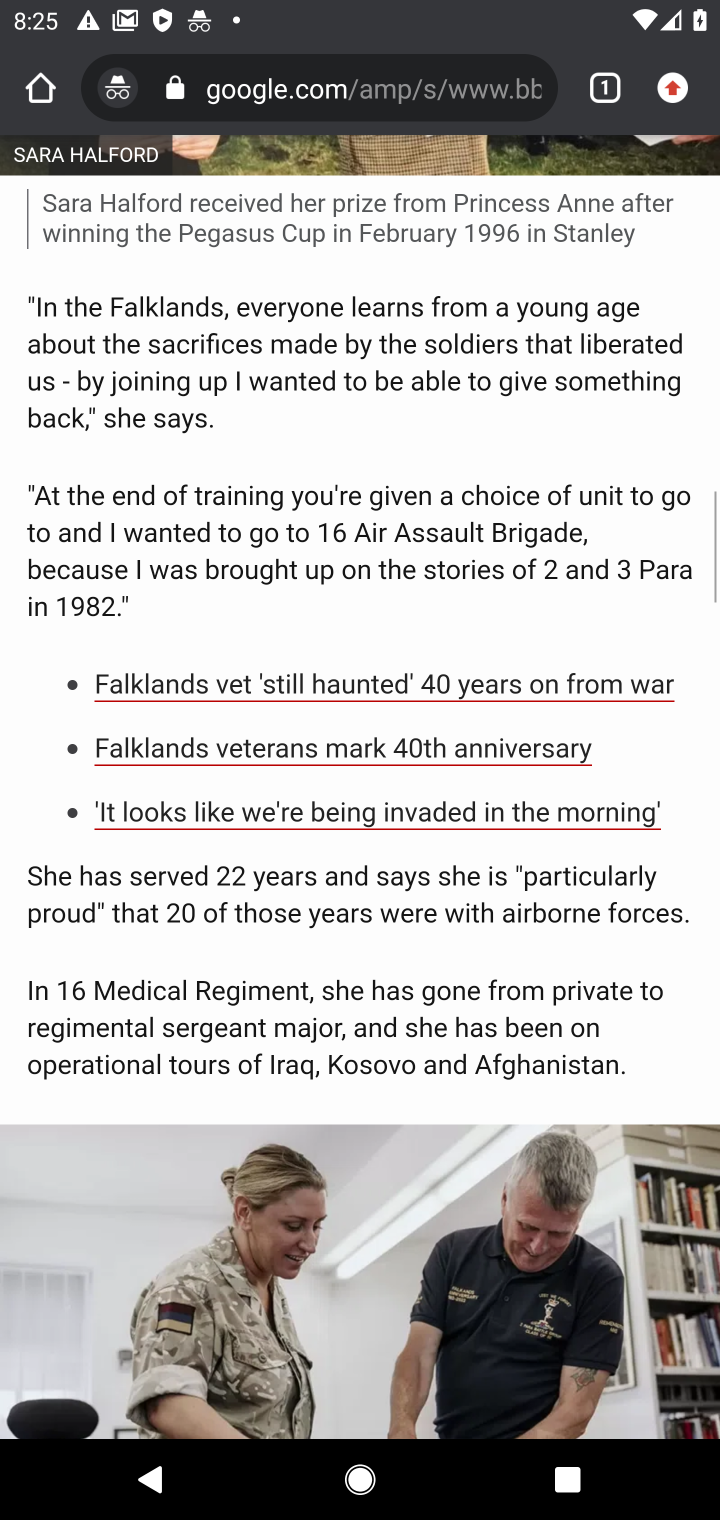
Step 59: drag from (423, 1268) to (485, 293)
Your task to perform on an android device: What's the news in theFalkland Islands? Image 60: 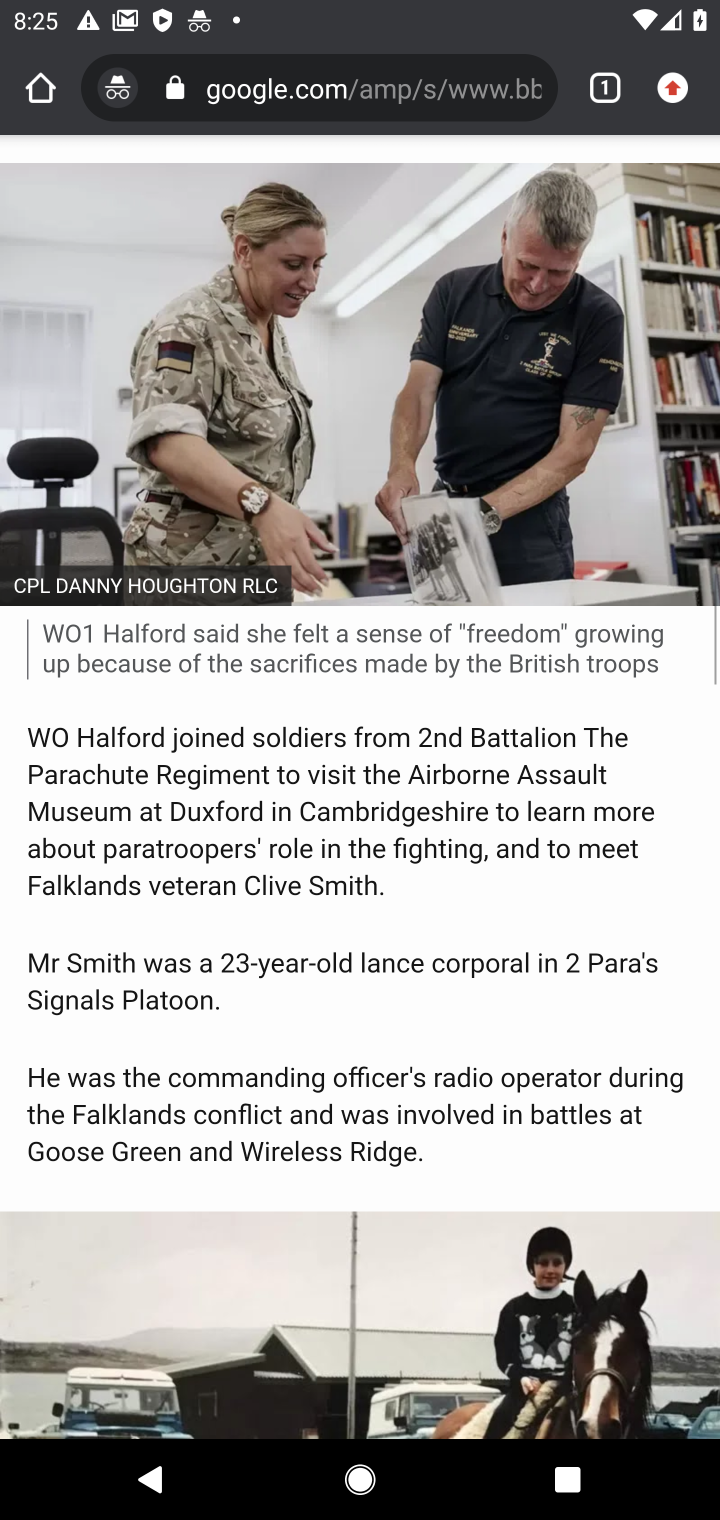
Step 60: drag from (442, 1027) to (473, 290)
Your task to perform on an android device: What's the news in theFalkland Islands? Image 61: 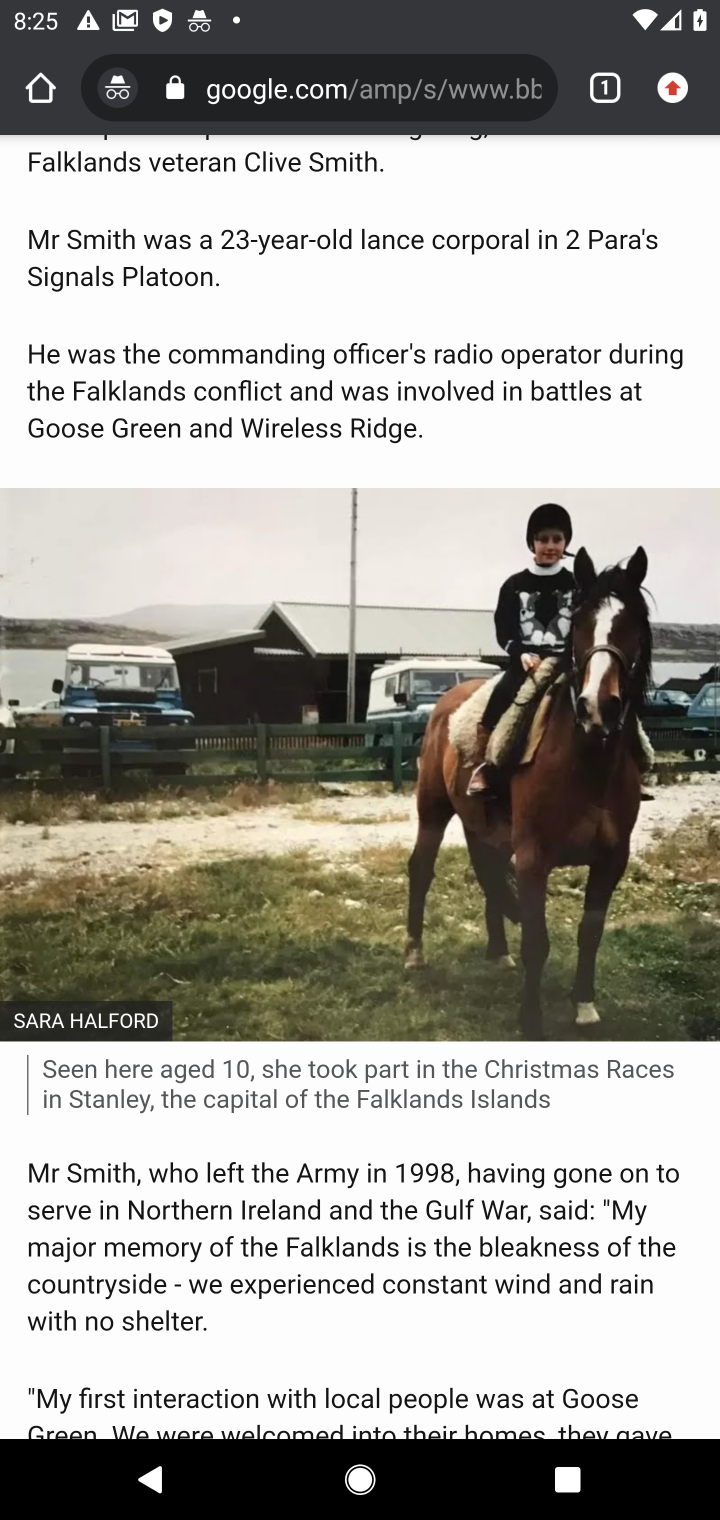
Step 61: drag from (488, 725) to (399, 317)
Your task to perform on an android device: What's the news in theFalkland Islands? Image 62: 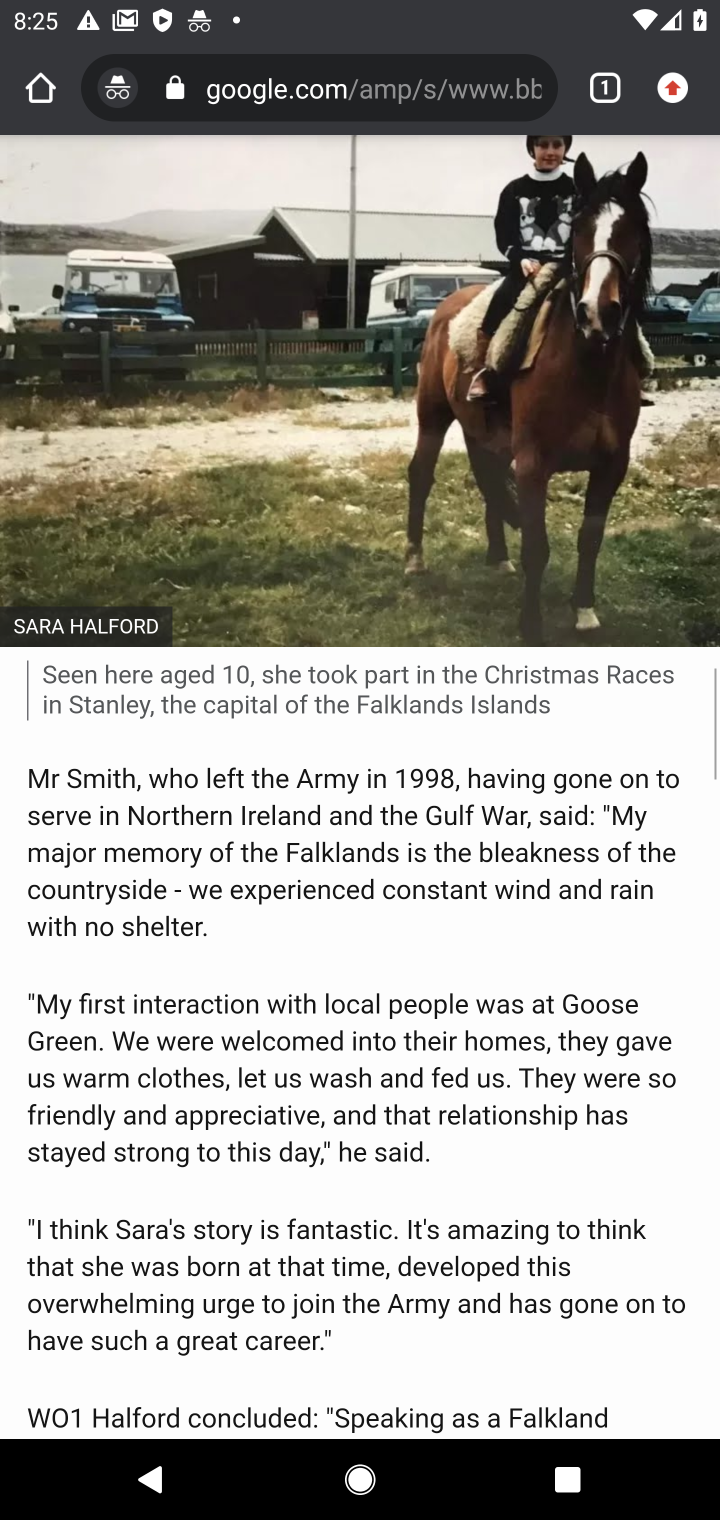
Step 62: press back button
Your task to perform on an android device: What's the news in theFalkland Islands? Image 63: 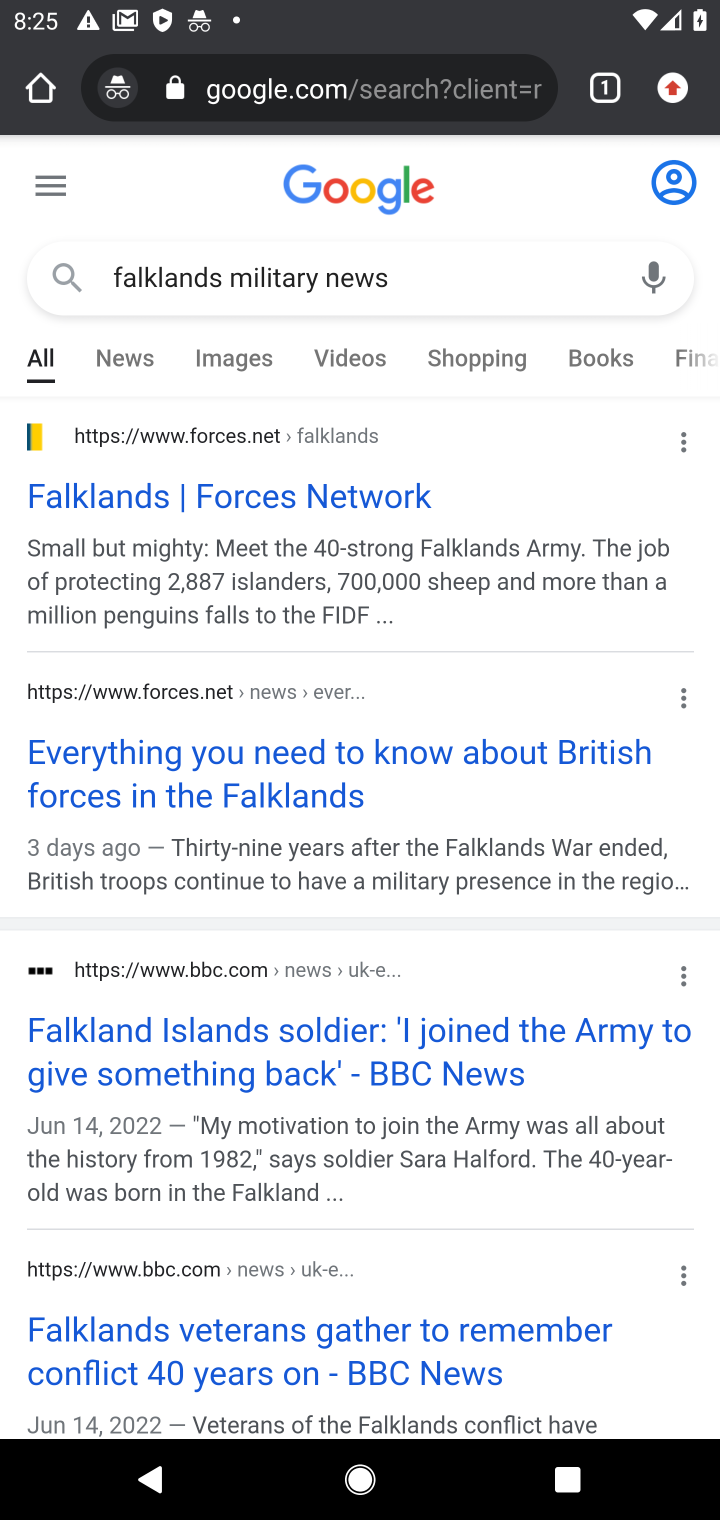
Step 63: click (265, 512)
Your task to perform on an android device: What's the news in theFalkland Islands? Image 64: 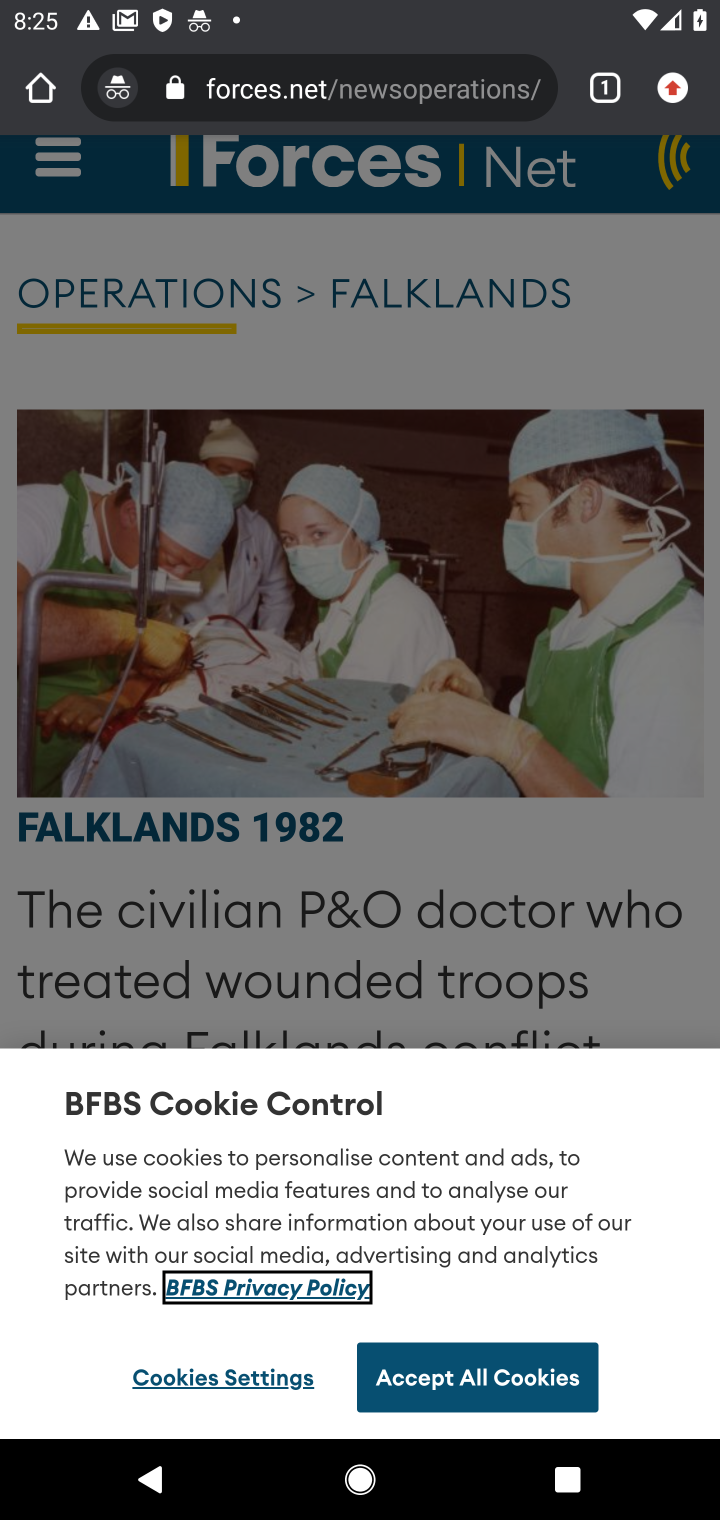
Step 64: click (226, 821)
Your task to perform on an android device: What's the news in theFalkland Islands? Image 65: 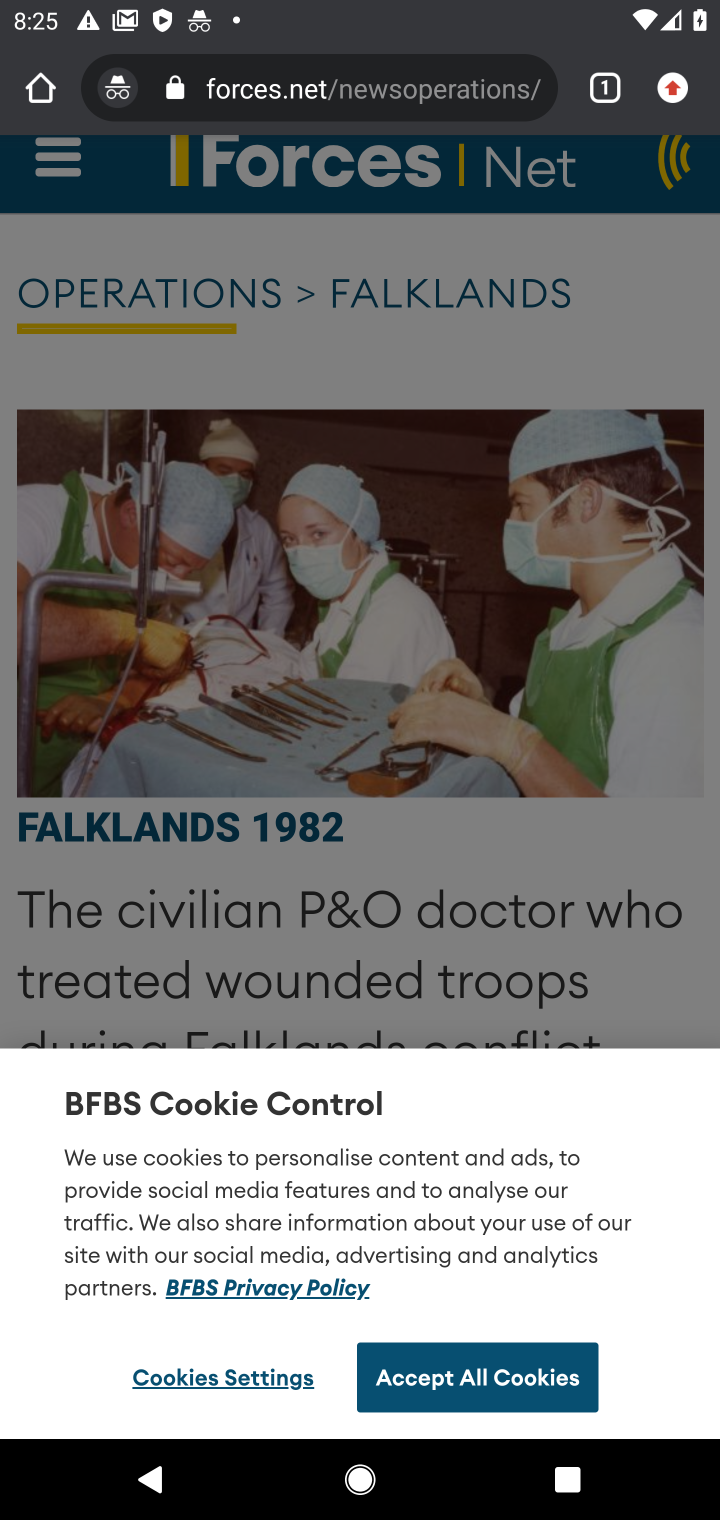
Step 65: click (508, 823)
Your task to perform on an android device: What's the news in theFalkland Islands? Image 66: 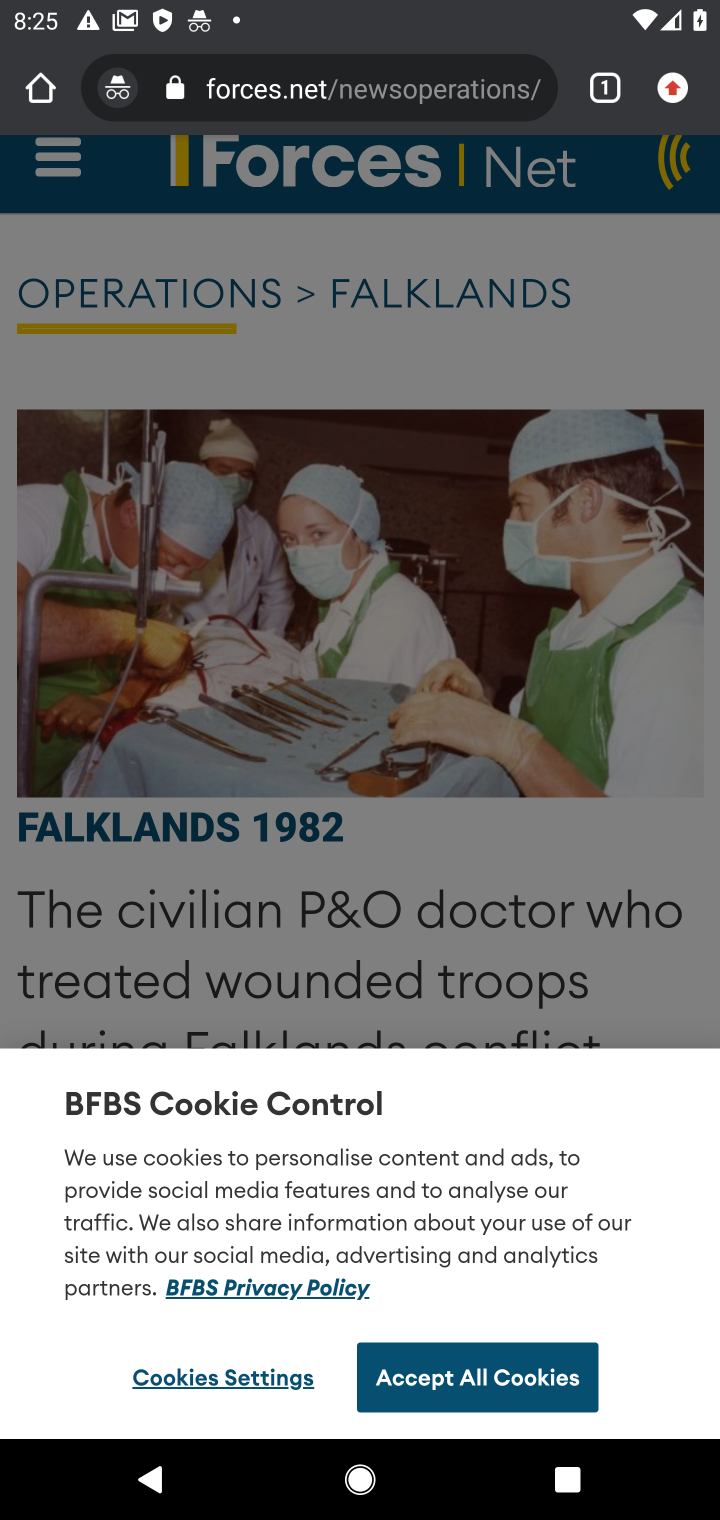
Step 66: drag from (533, 899) to (582, 270)
Your task to perform on an android device: What's the news in theFalkland Islands? Image 67: 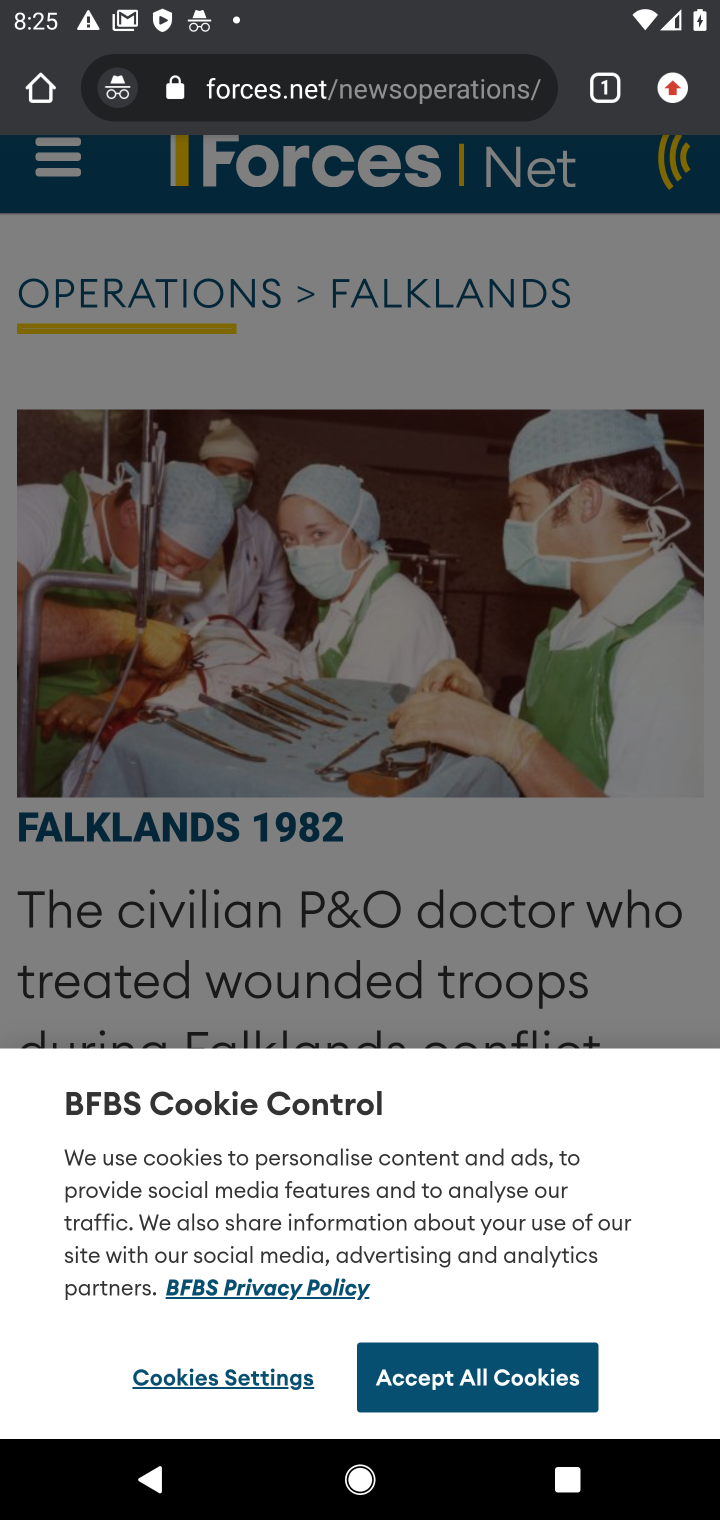
Step 67: click (408, 929)
Your task to perform on an android device: What's the news in theFalkland Islands? Image 68: 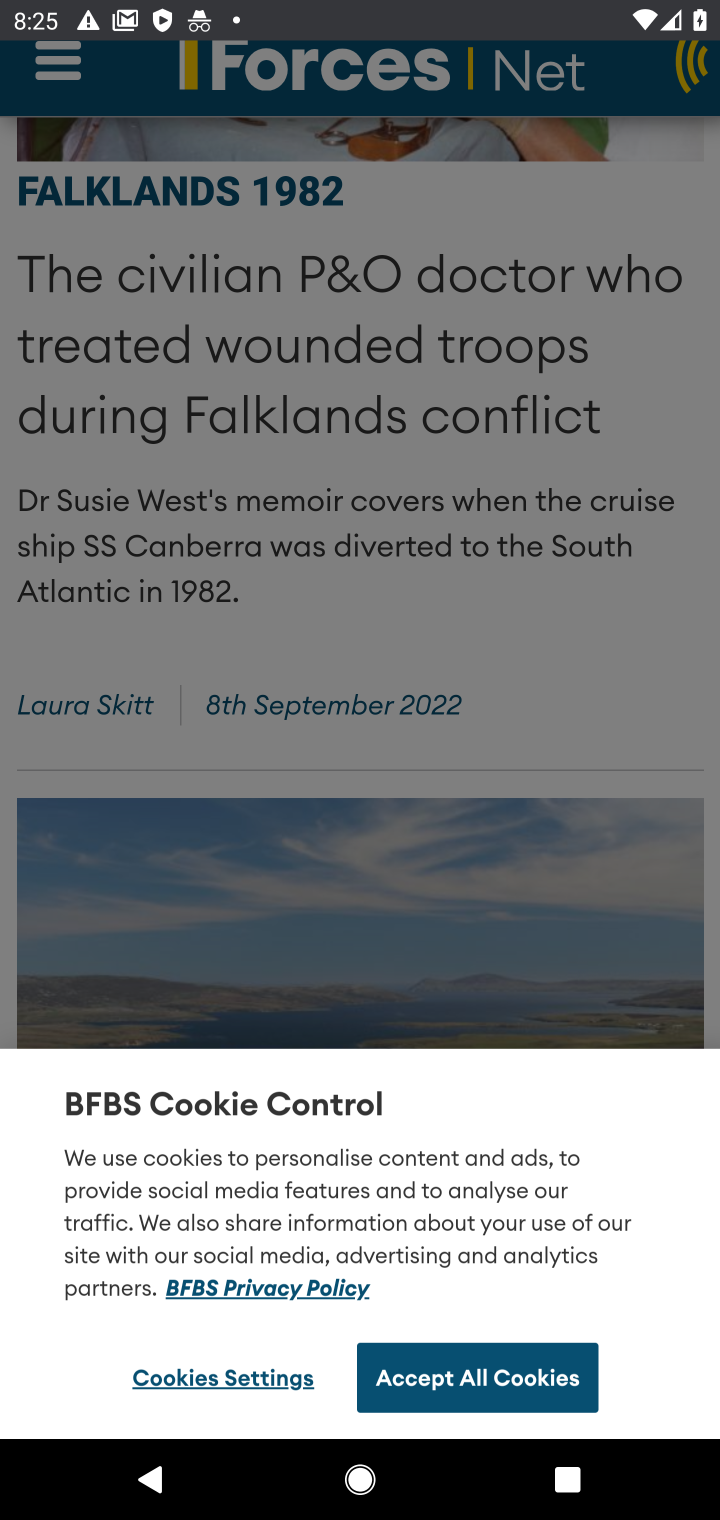
Step 68: click (471, 1357)
Your task to perform on an android device: What's the news in theFalkland Islands? Image 69: 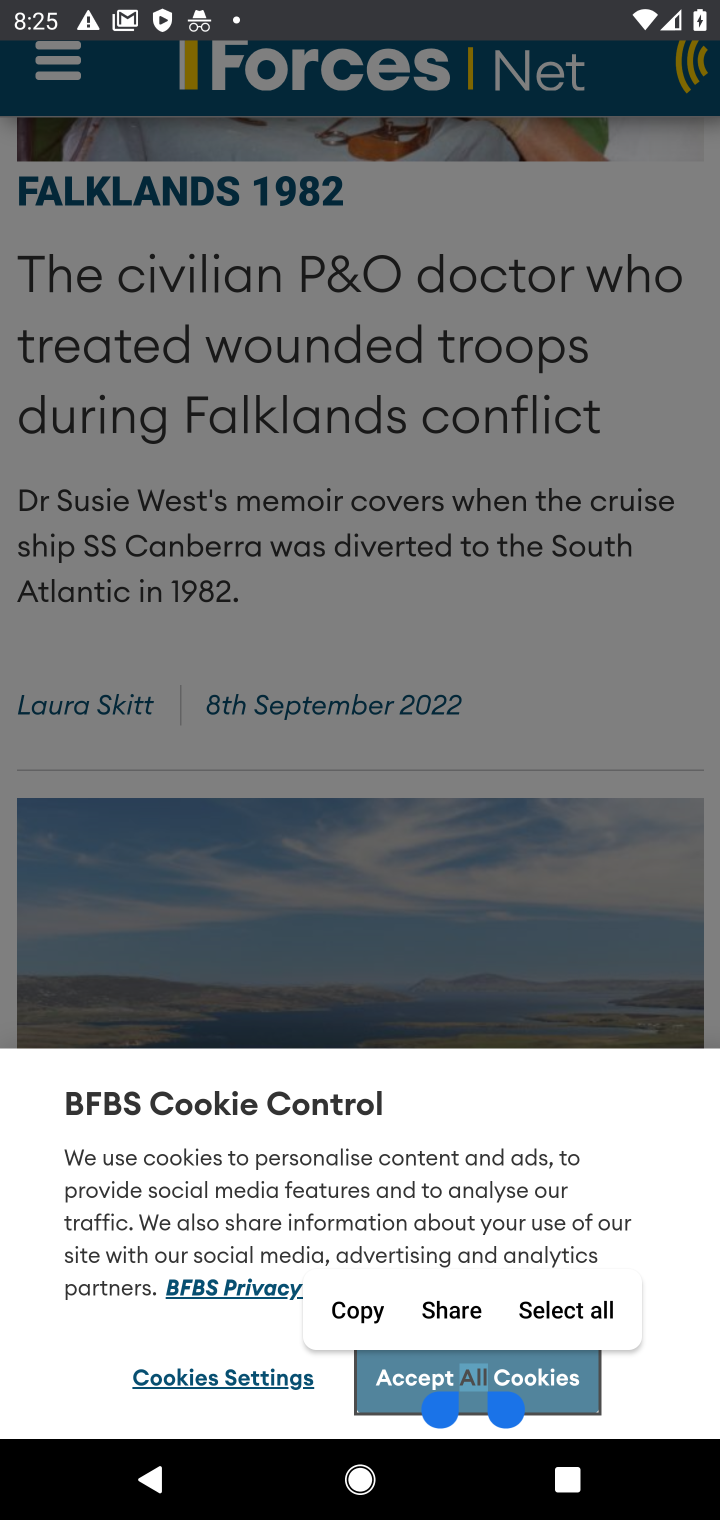
Step 69: click (517, 850)
Your task to perform on an android device: What's the news in theFalkland Islands? Image 70: 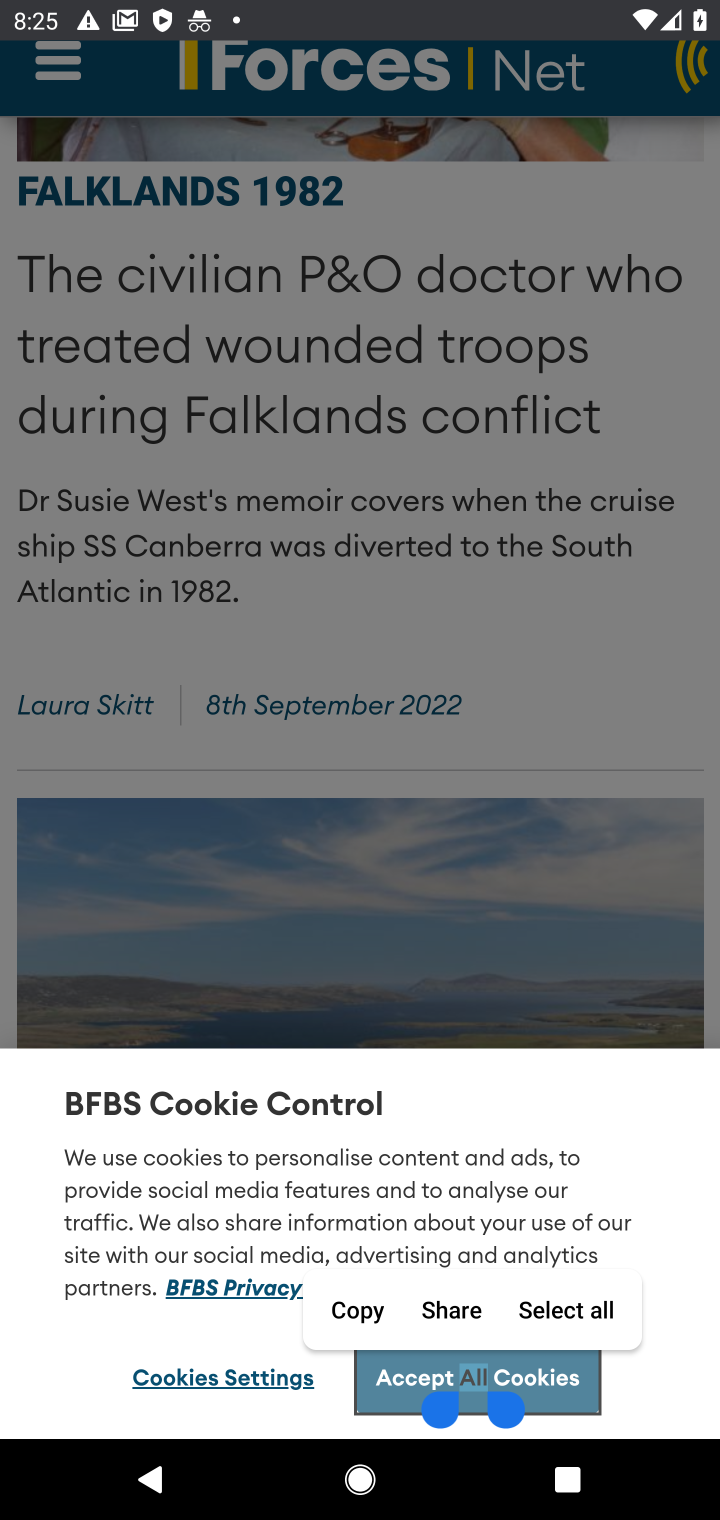
Step 70: click (518, 1390)
Your task to perform on an android device: What's the news in theFalkland Islands? Image 71: 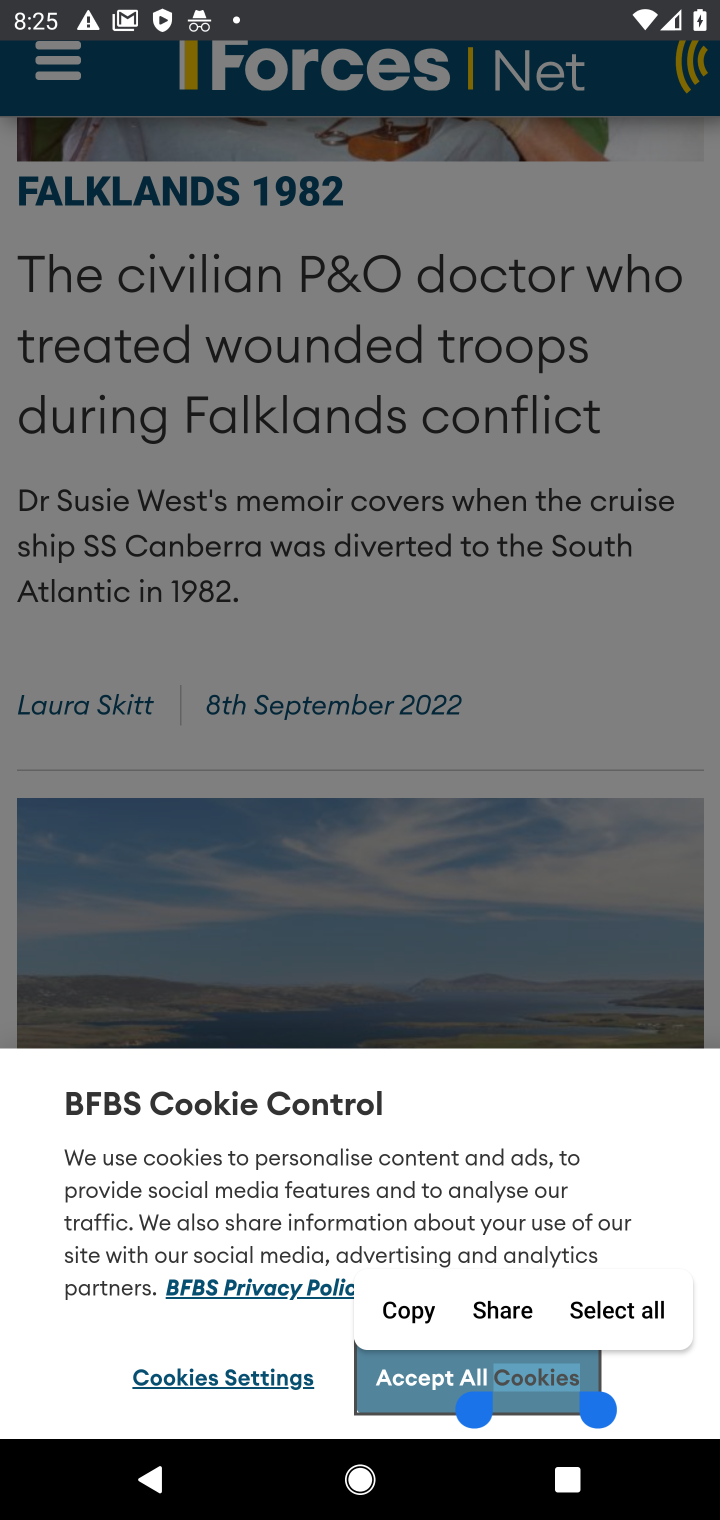
Step 71: click (457, 1390)
Your task to perform on an android device: What's the news in theFalkland Islands? Image 72: 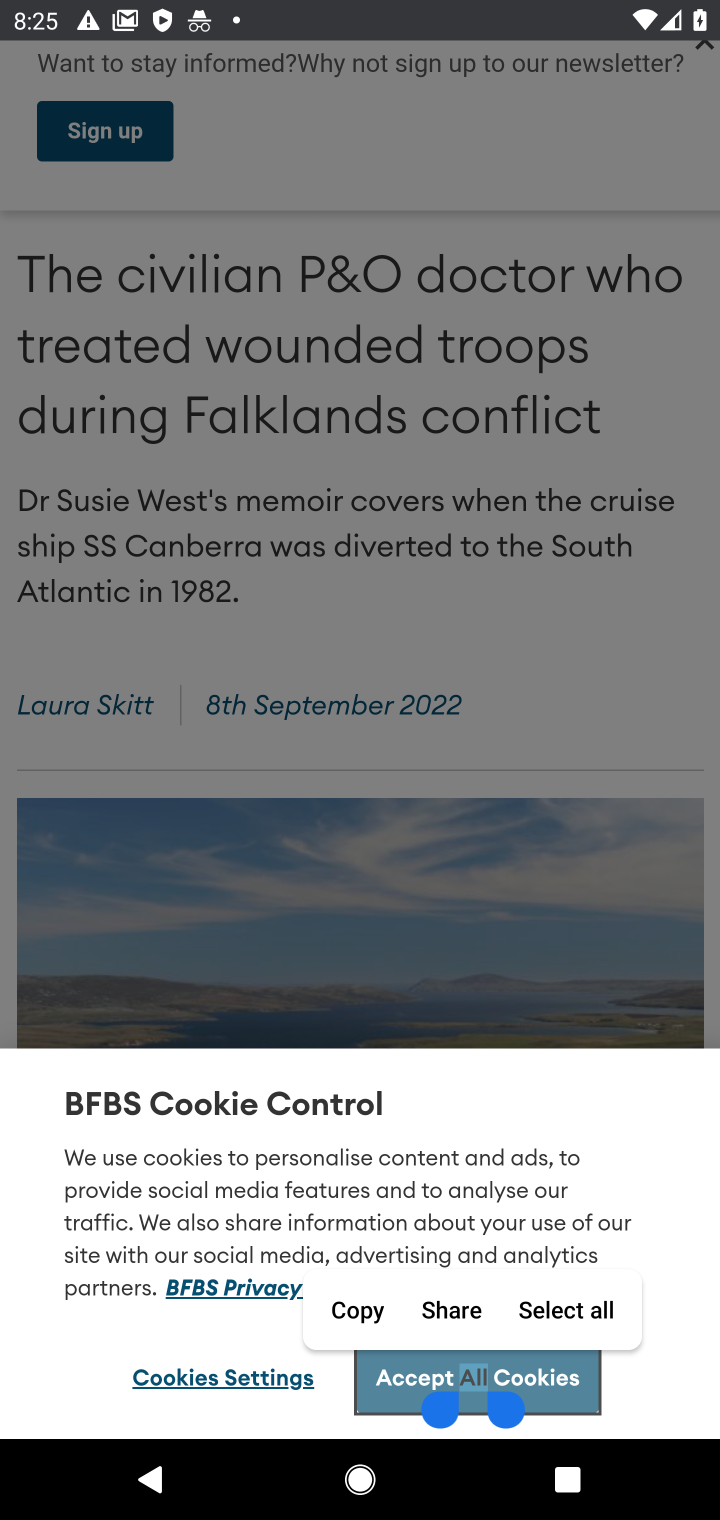
Step 72: click (404, 718)
Your task to perform on an android device: What's the news in theFalkland Islands? Image 73: 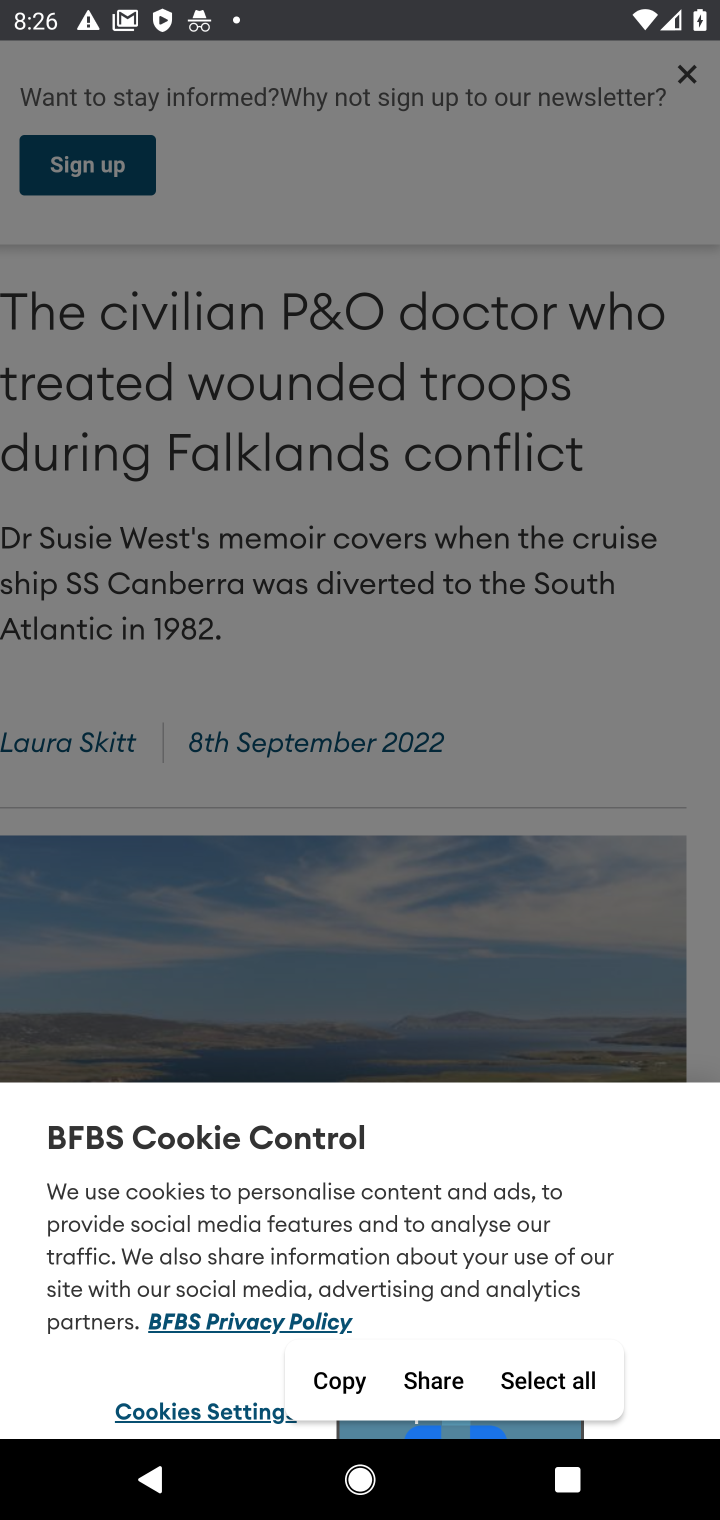
Step 73: click (374, 1420)
Your task to perform on an android device: What's the news in theFalkland Islands? Image 74: 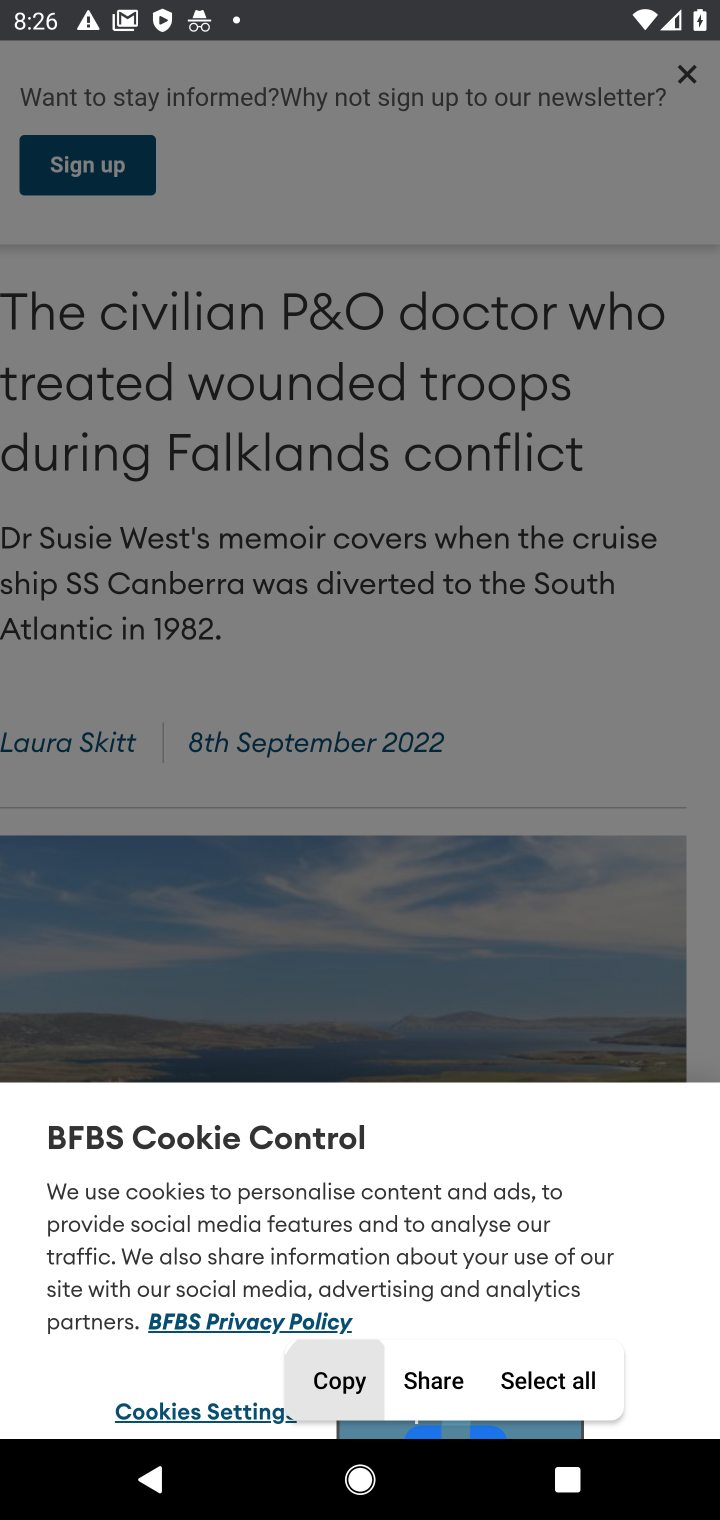
Step 74: drag from (585, 752) to (555, 524)
Your task to perform on an android device: What's the news in theFalkland Islands? Image 75: 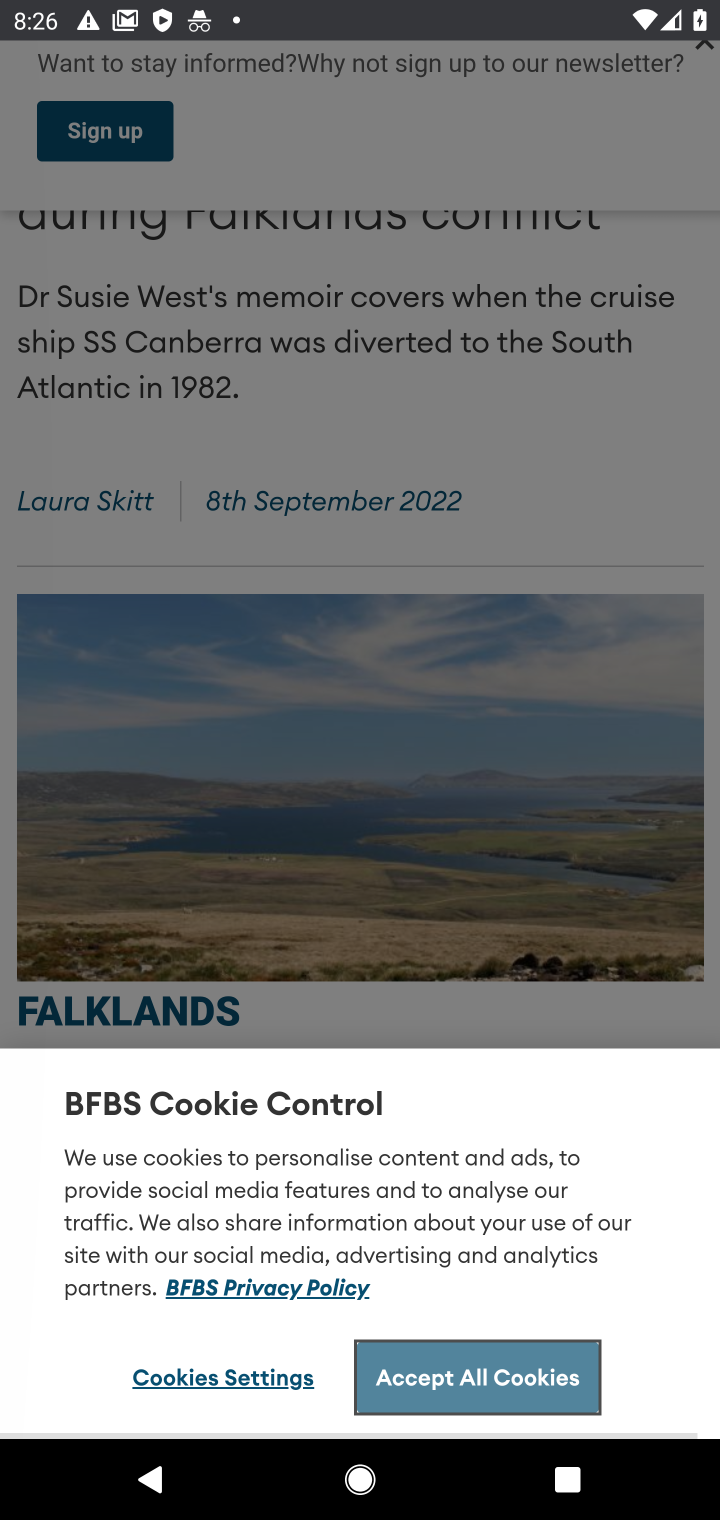
Step 75: click (402, 1410)
Your task to perform on an android device: What's the news in theFalkland Islands? Image 76: 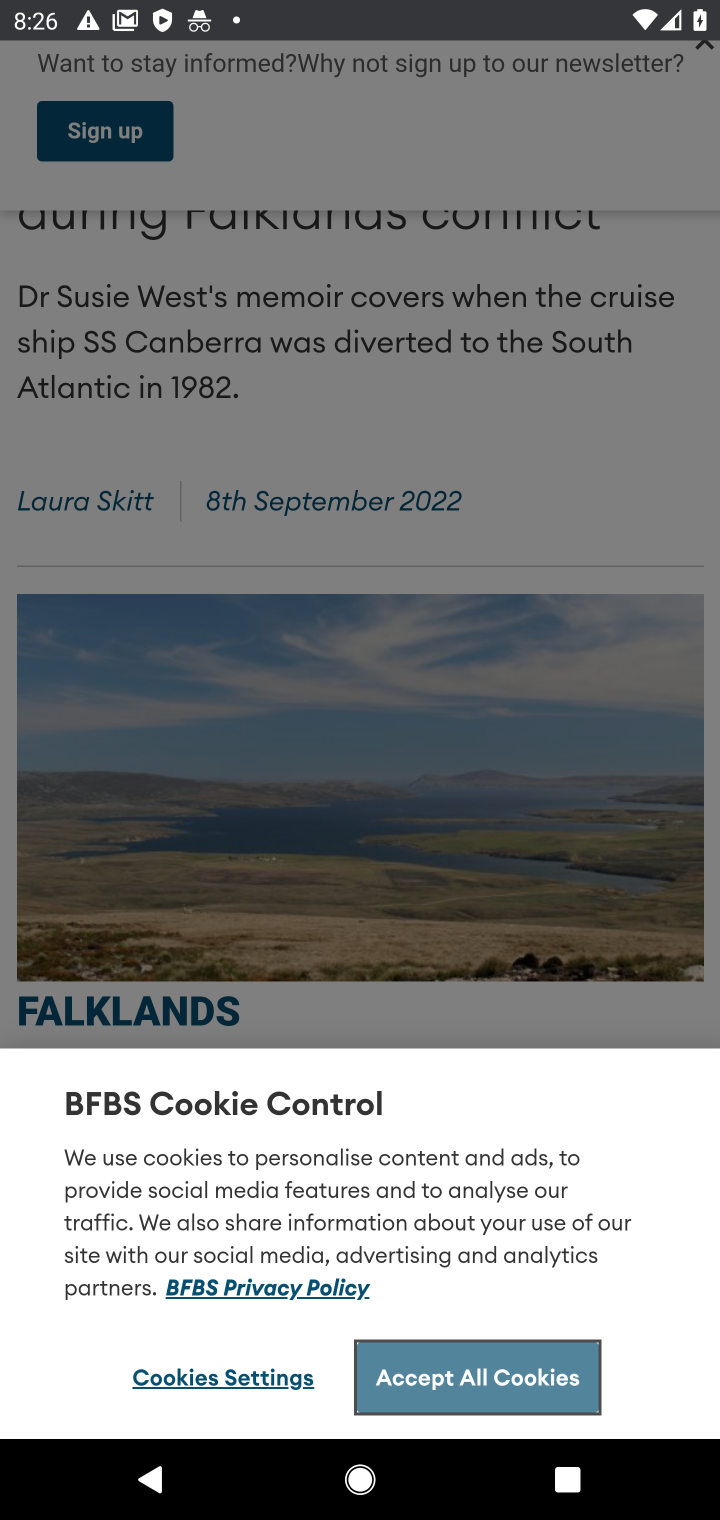
Step 76: task complete